Your task to perform on an android device: What's the news in India? Image 0: 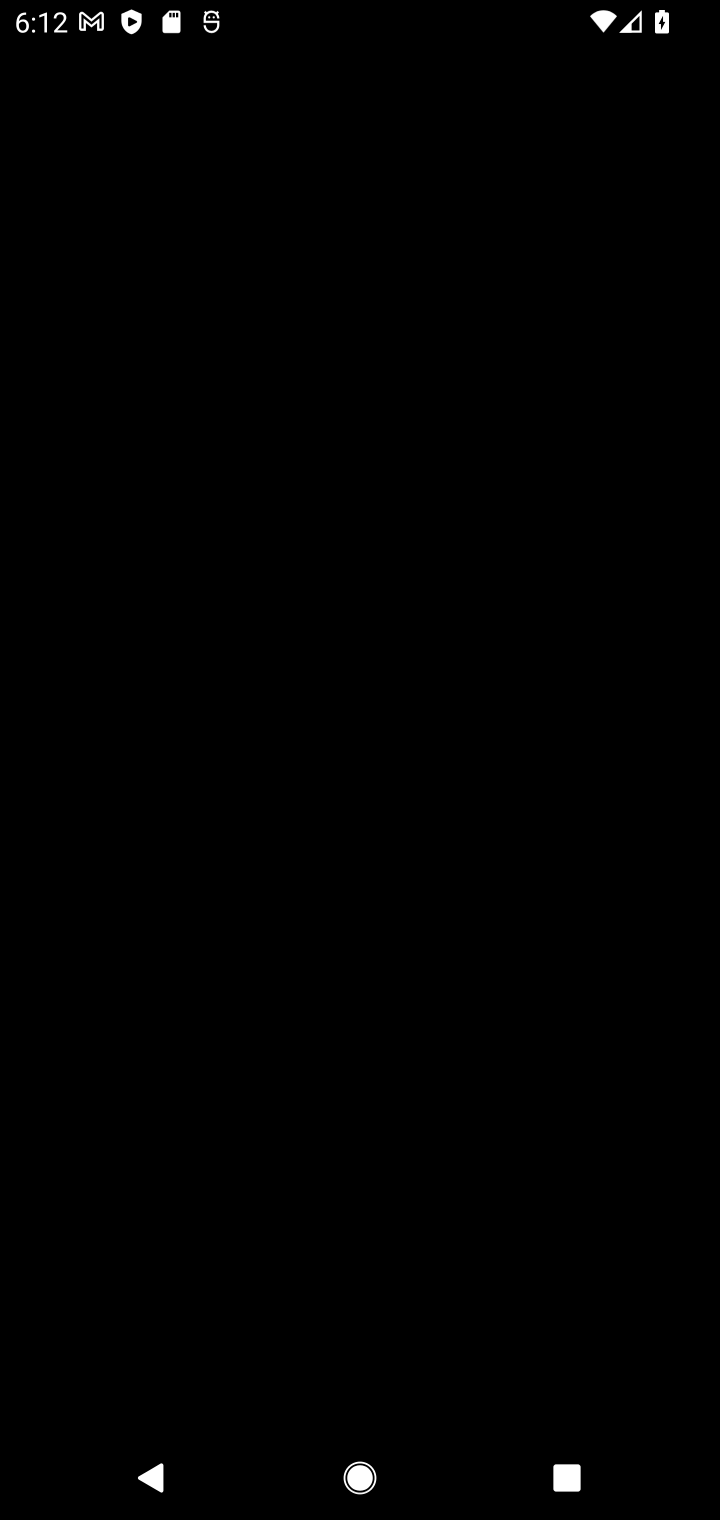
Step 0: press home button
Your task to perform on an android device: What's the news in India? Image 1: 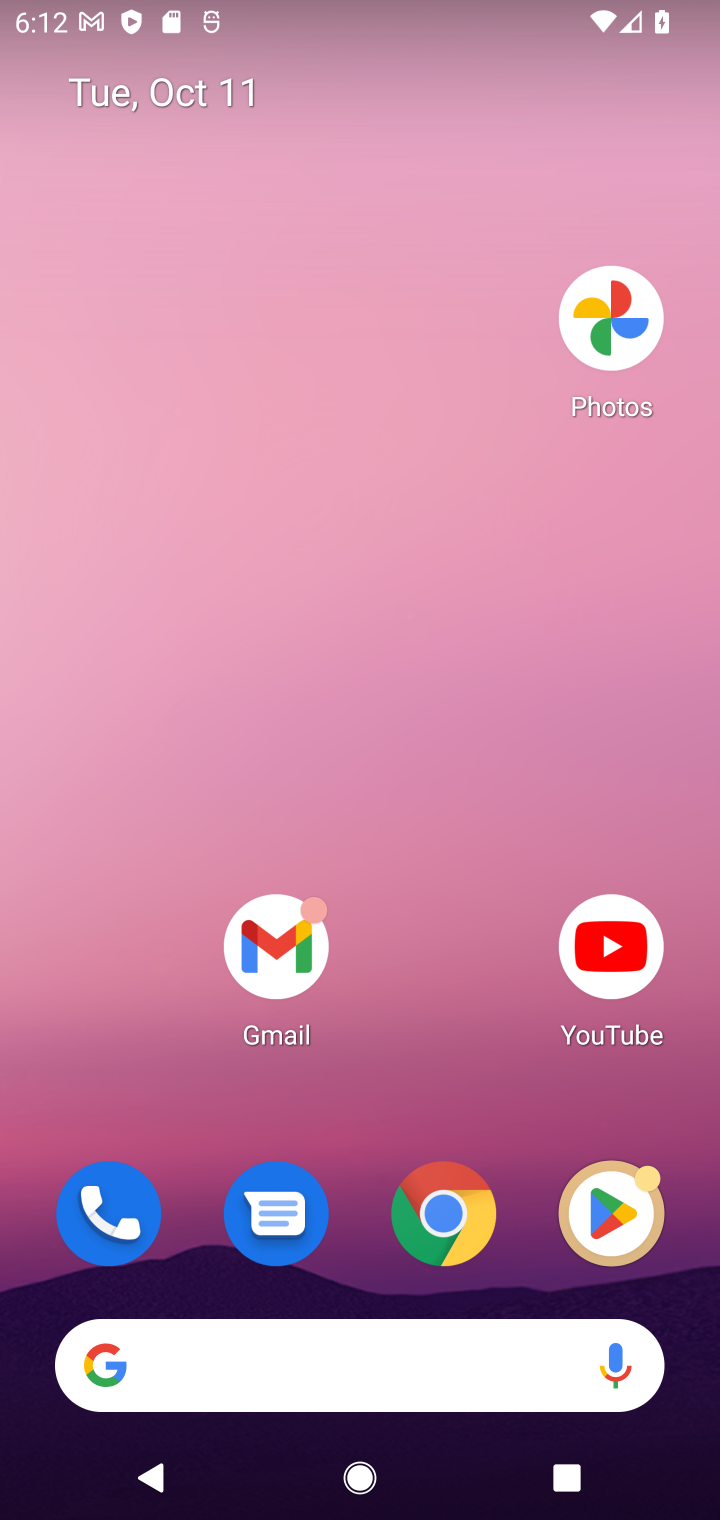
Step 1: drag from (382, 1139) to (526, 72)
Your task to perform on an android device: What's the news in India? Image 2: 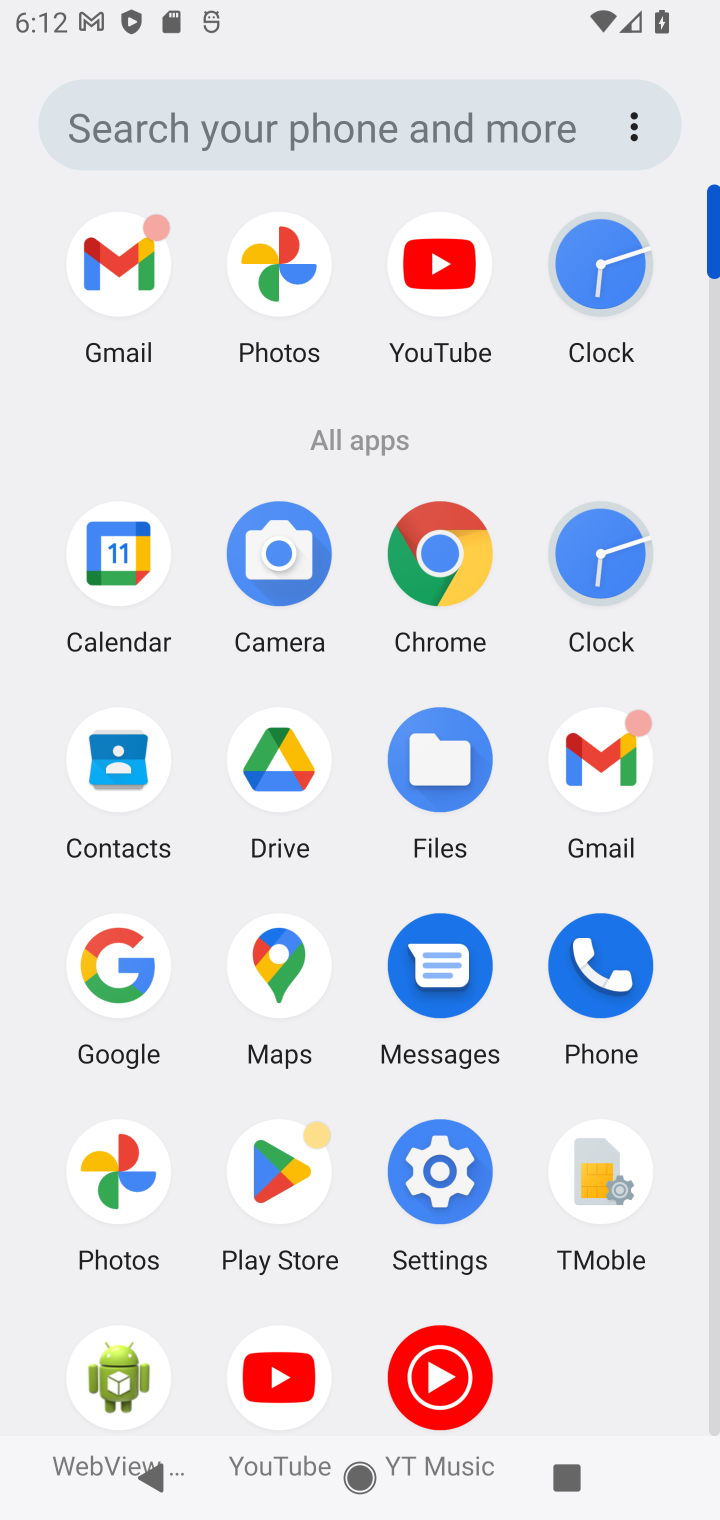
Step 2: click (441, 554)
Your task to perform on an android device: What's the news in India? Image 3: 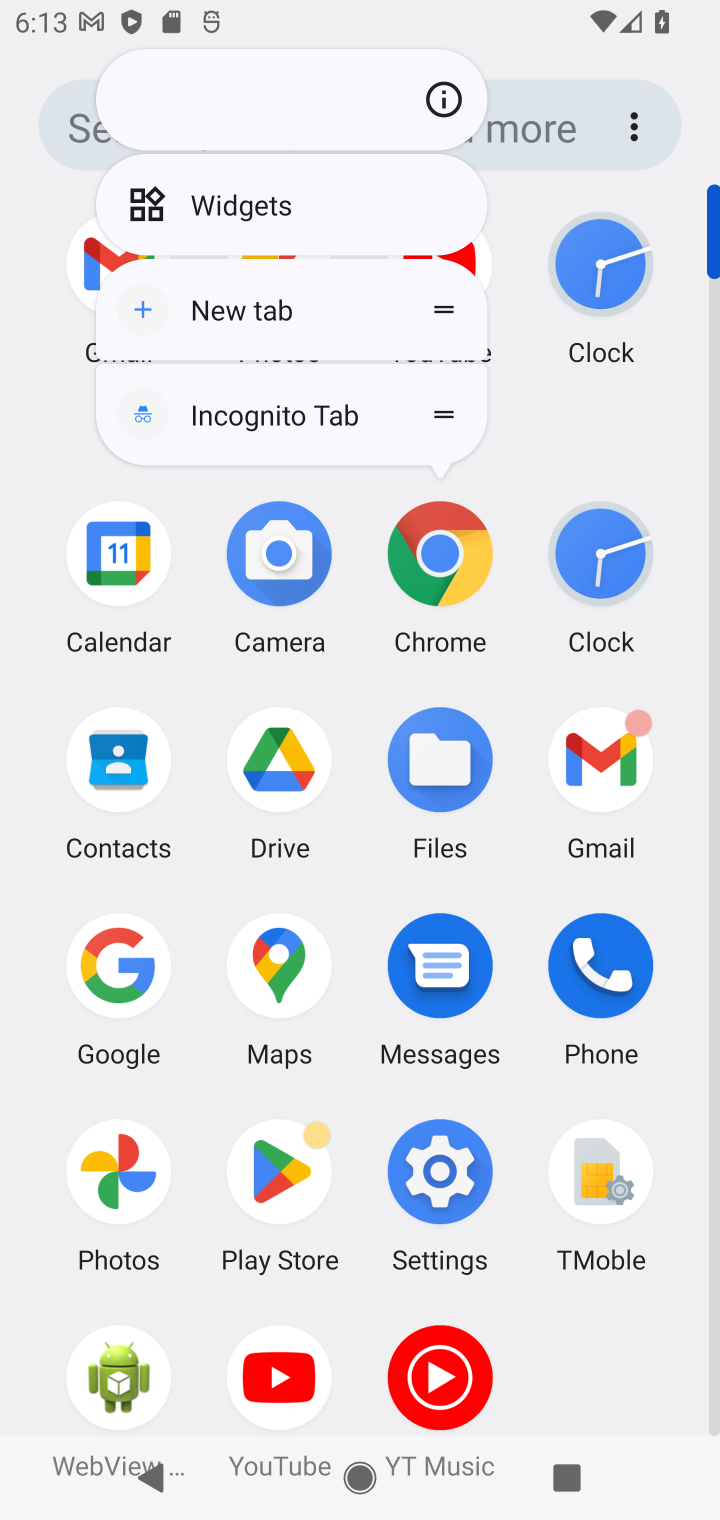
Step 3: click (436, 572)
Your task to perform on an android device: What's the news in India? Image 4: 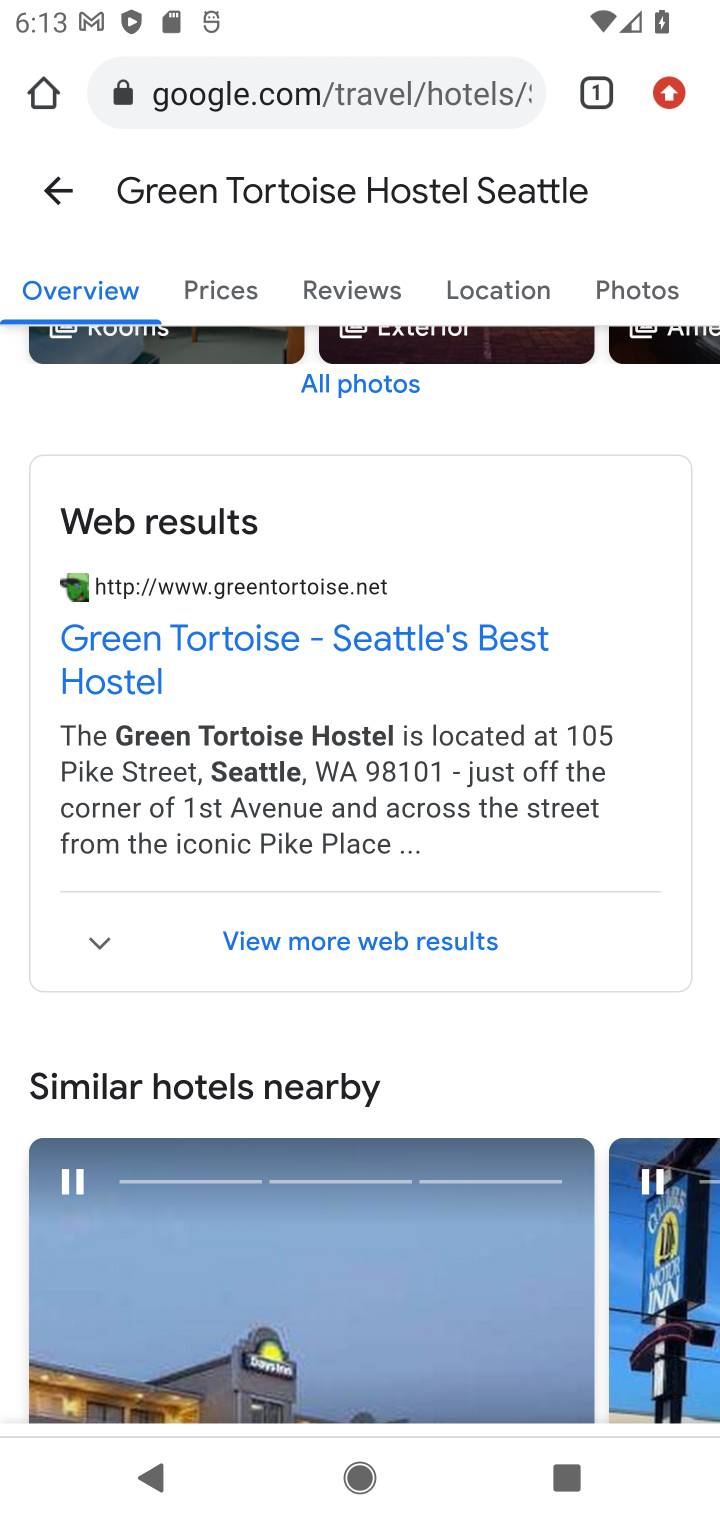
Step 4: click (378, 83)
Your task to perform on an android device: What's the news in India? Image 5: 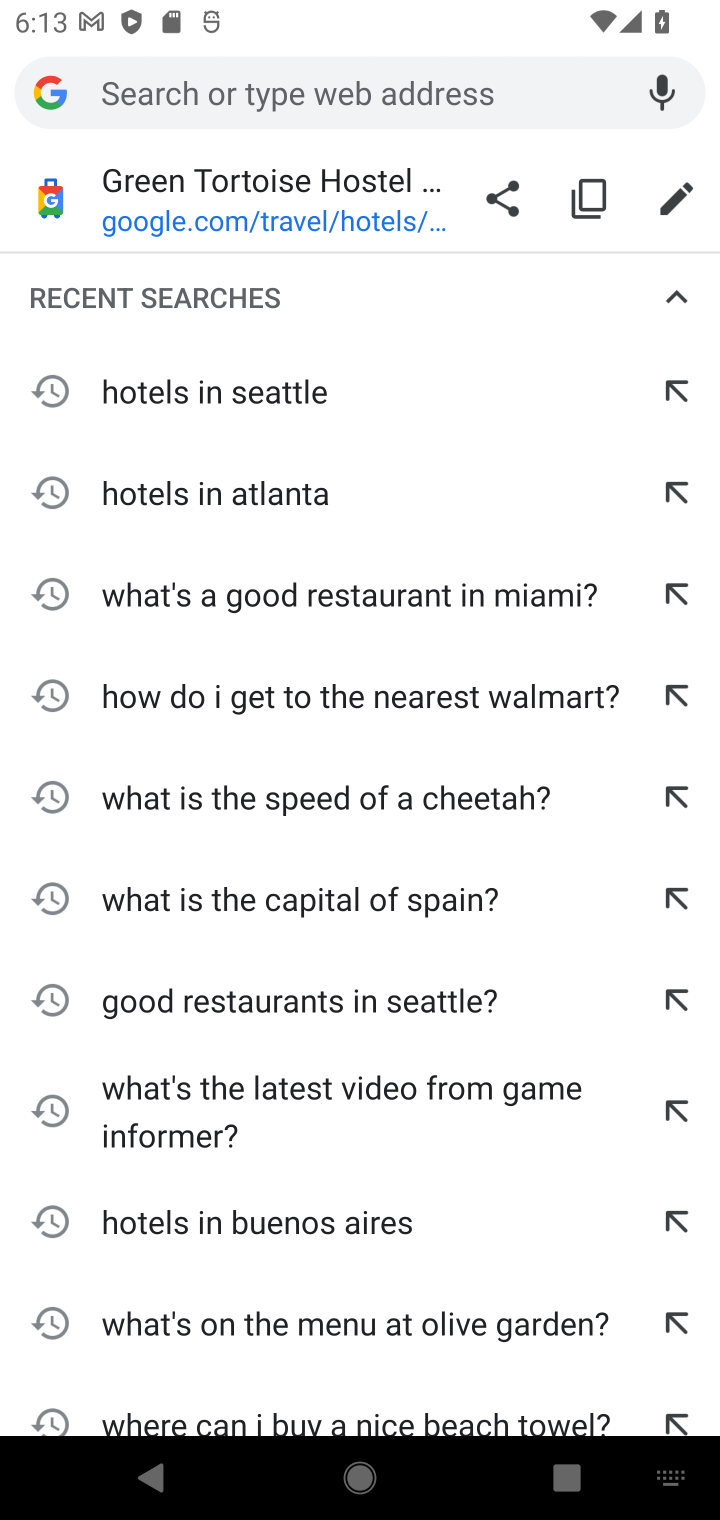
Step 5: type "hotels in Seattle"
Your task to perform on an android device: What's the news in India? Image 6: 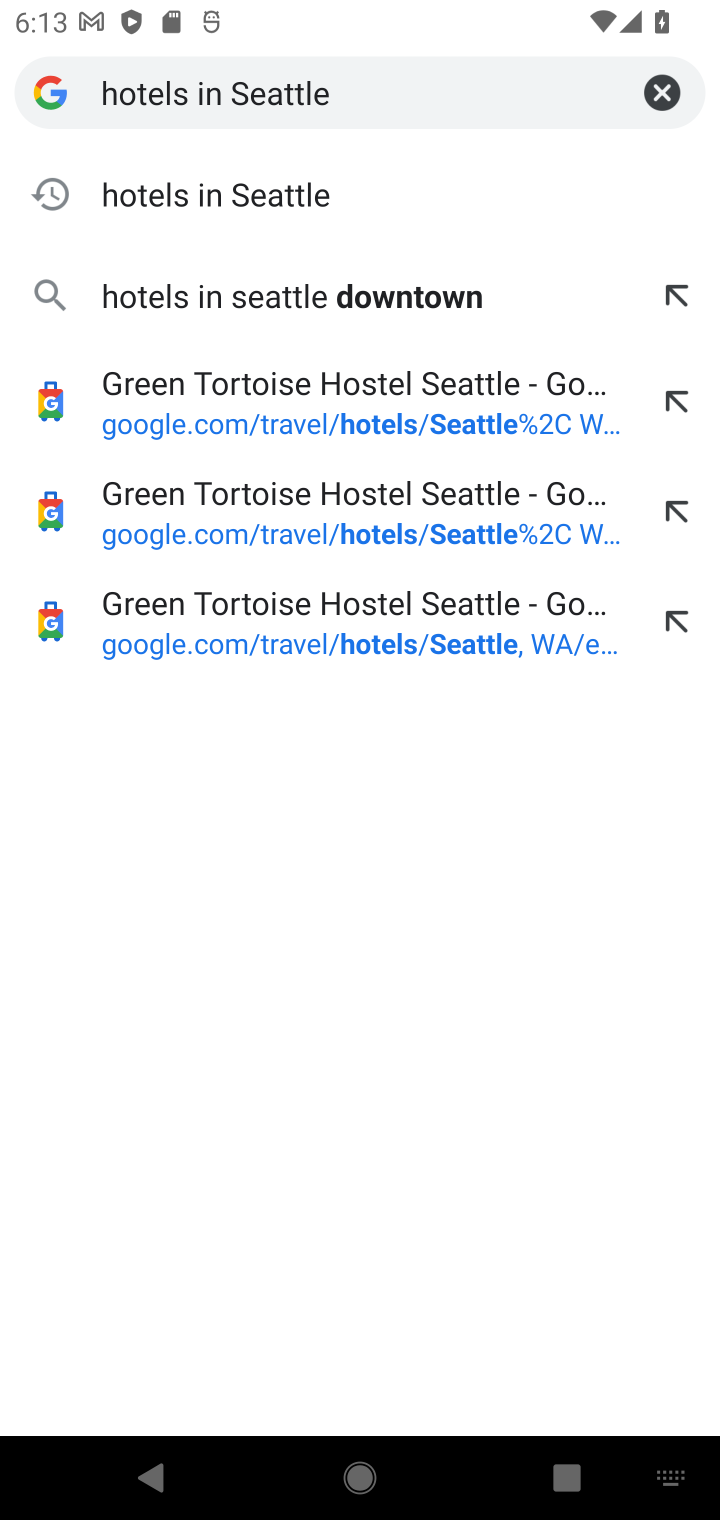
Step 6: press enter
Your task to perform on an android device: What's the news in India? Image 7: 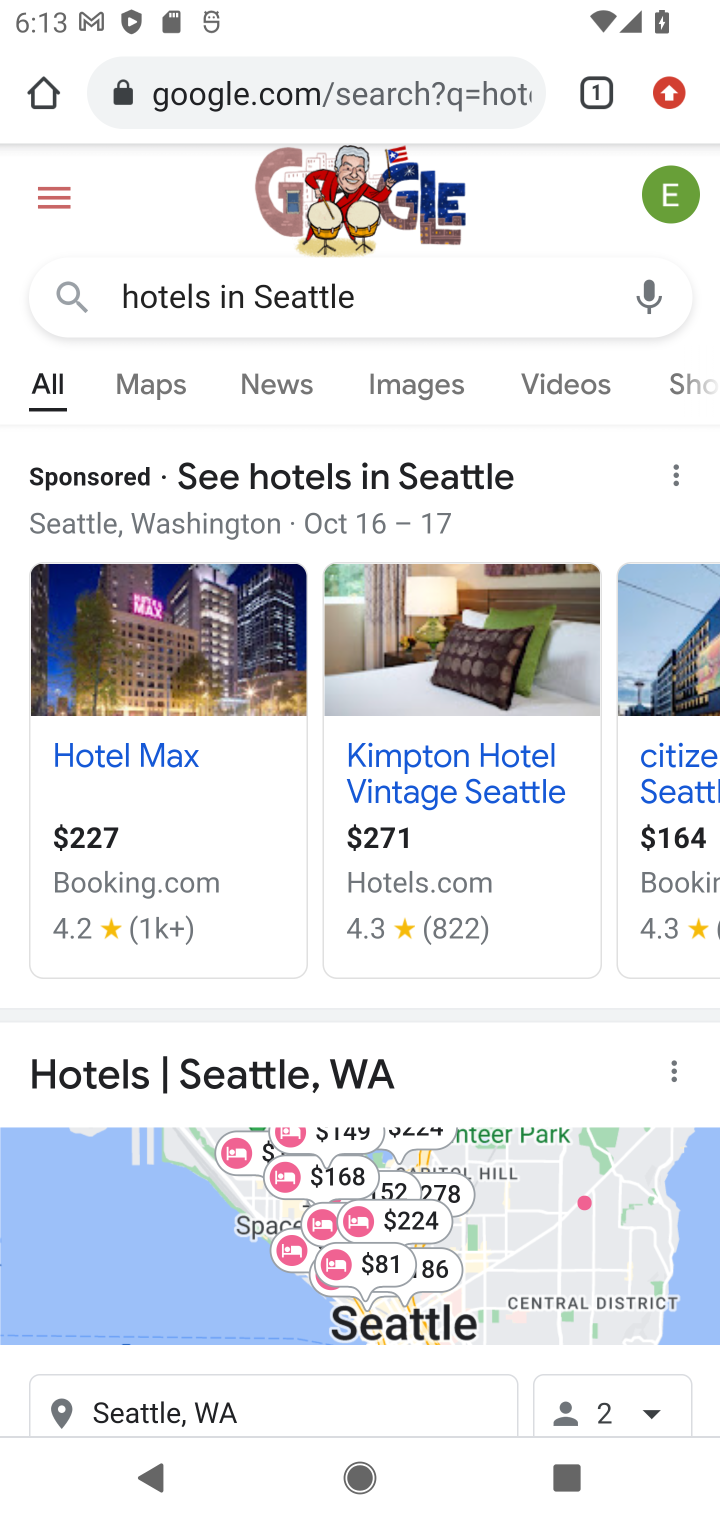
Step 7: click (491, 89)
Your task to perform on an android device: What's the news in India? Image 8: 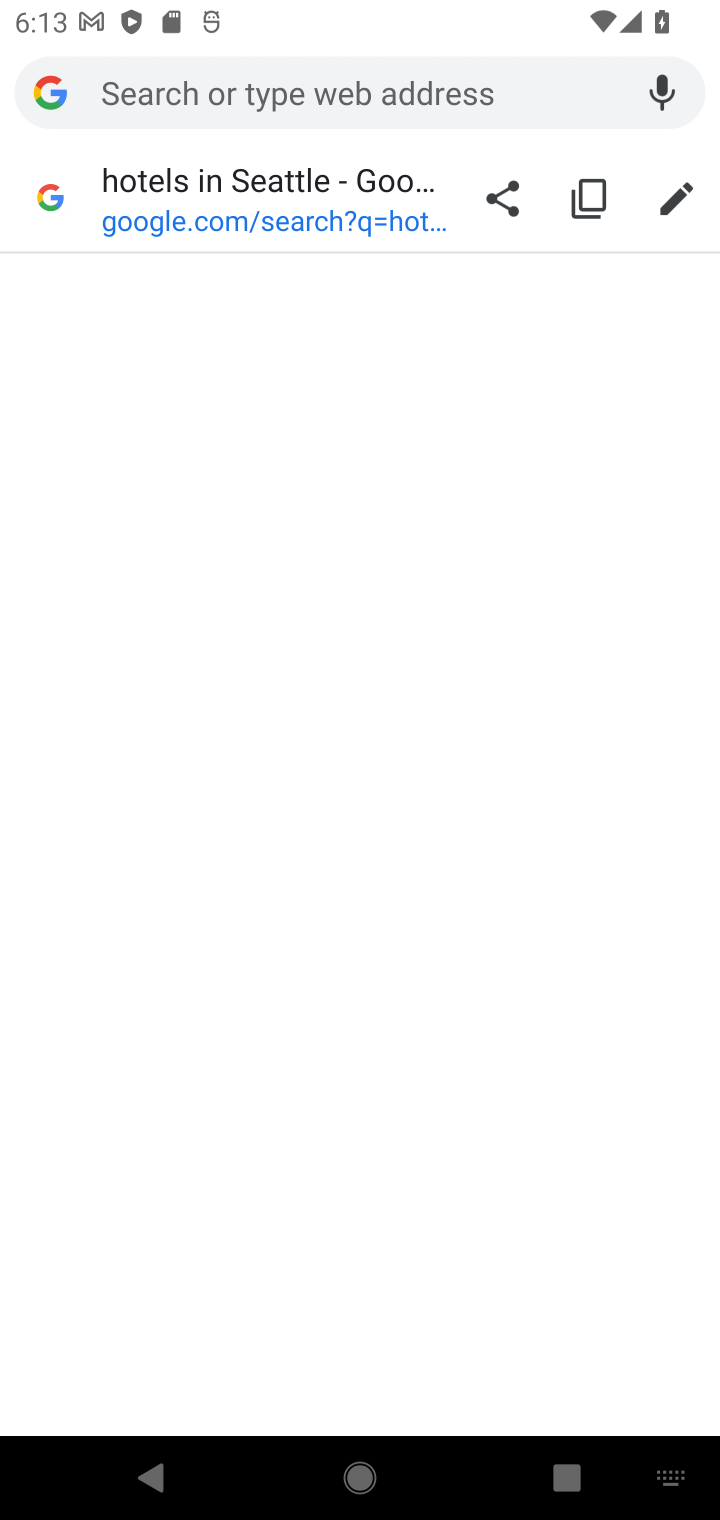
Step 8: type "What's the news in India?"
Your task to perform on an android device: What's the news in India? Image 9: 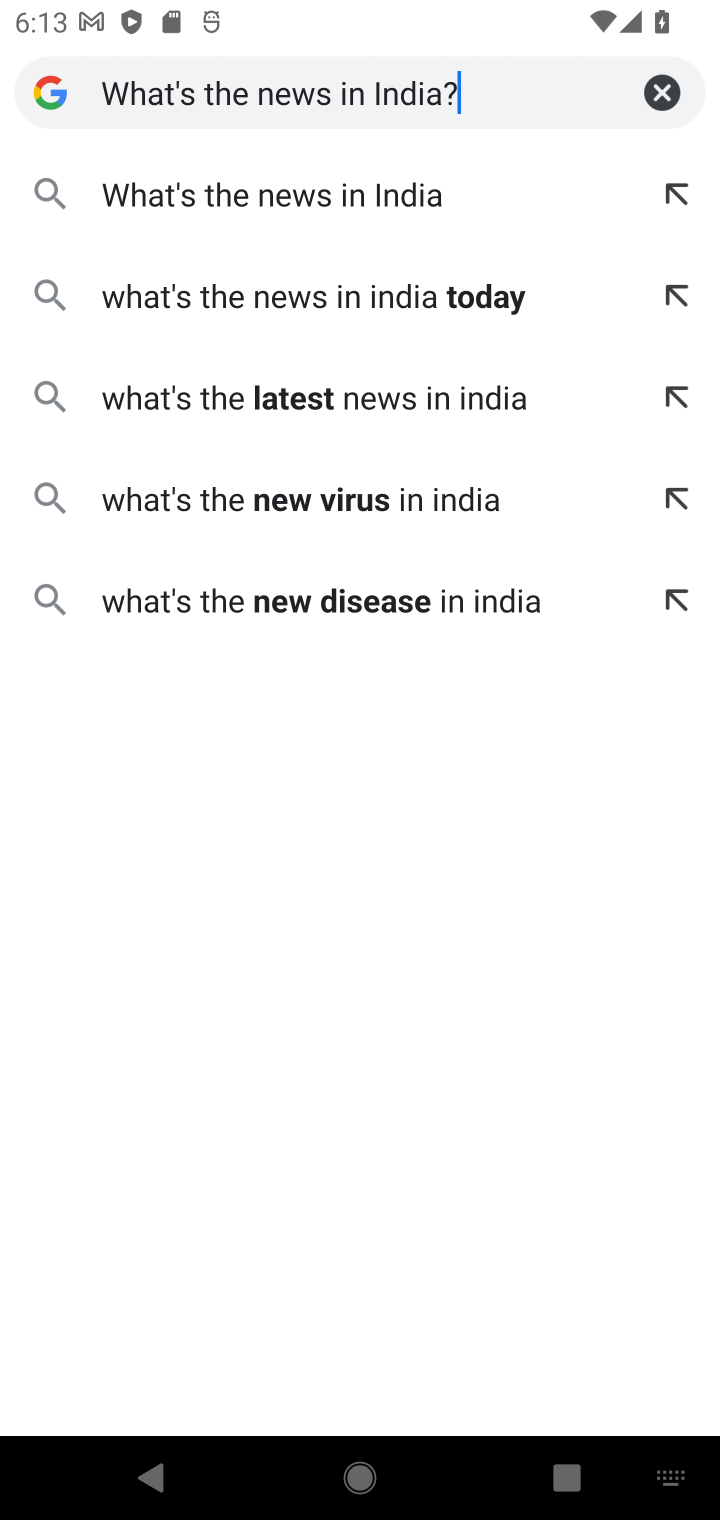
Step 9: type ""
Your task to perform on an android device: What's the news in India? Image 10: 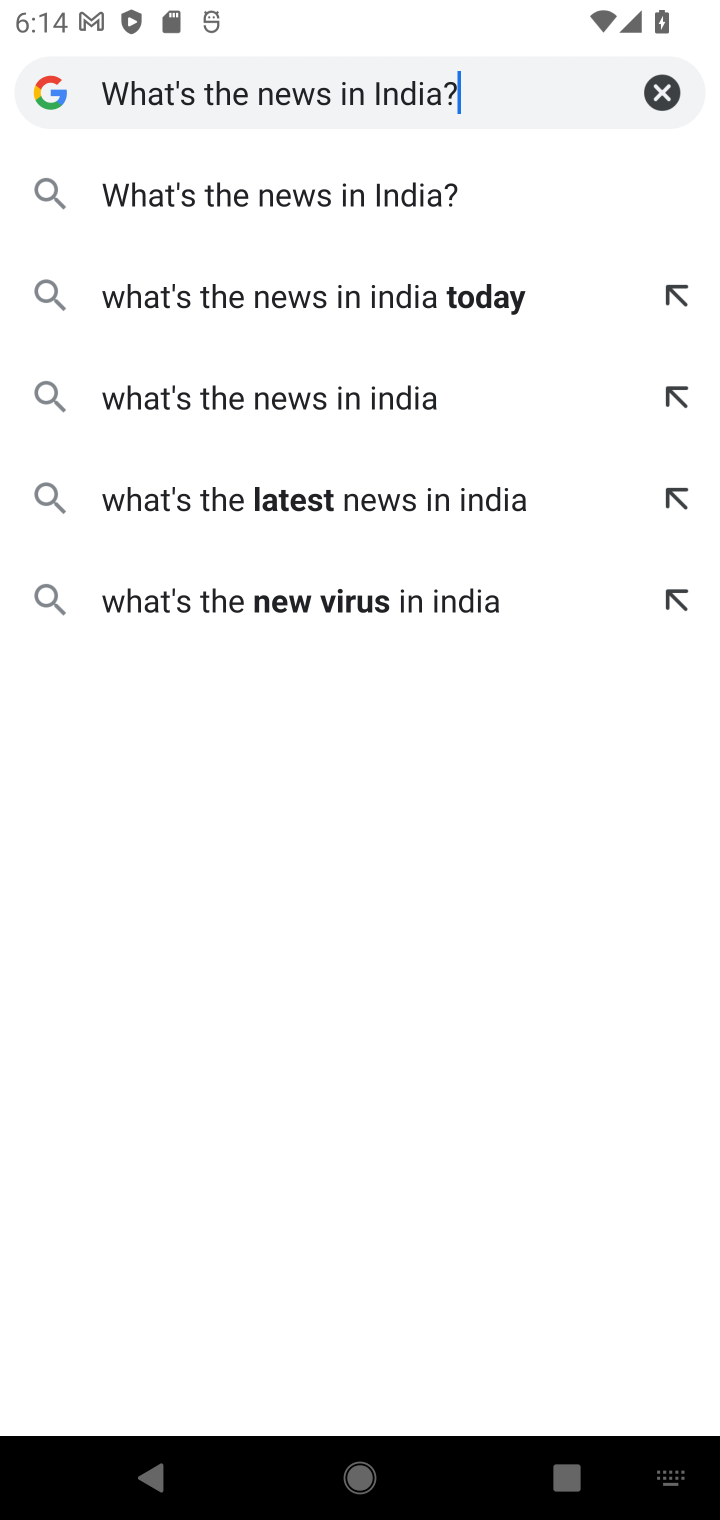
Step 10: click (334, 223)
Your task to perform on an android device: What's the news in India? Image 11: 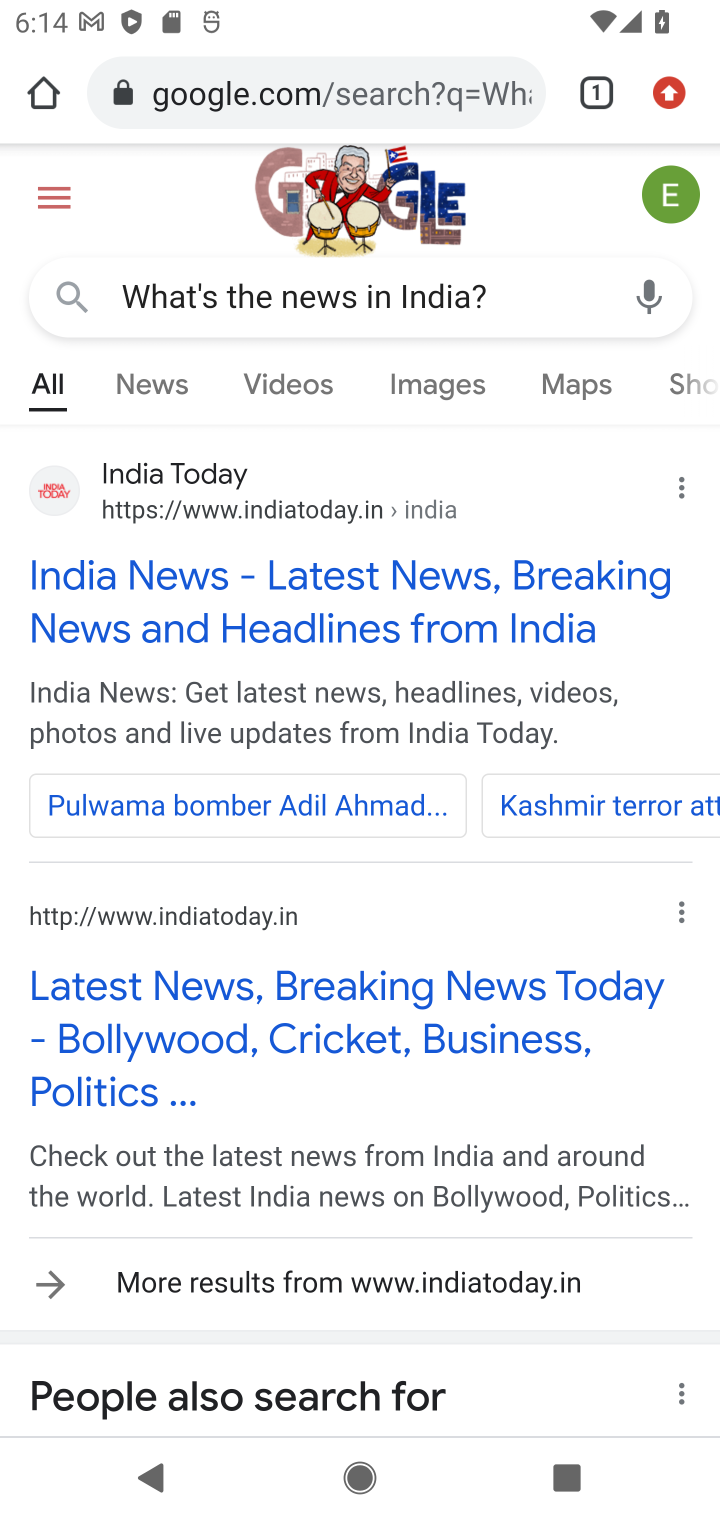
Step 11: click (173, 585)
Your task to perform on an android device: What's the news in India? Image 12: 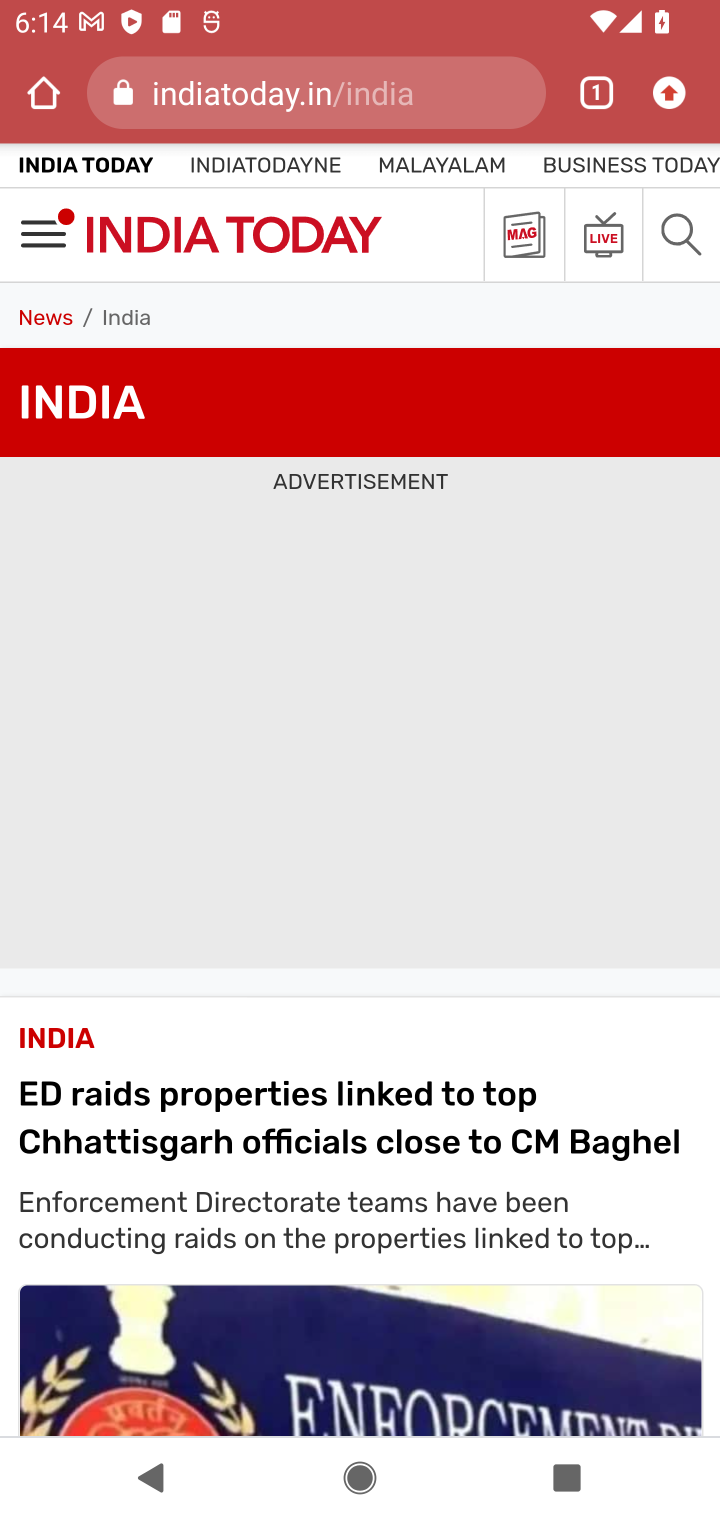
Step 12: drag from (153, 1277) to (125, 456)
Your task to perform on an android device: What's the news in India? Image 13: 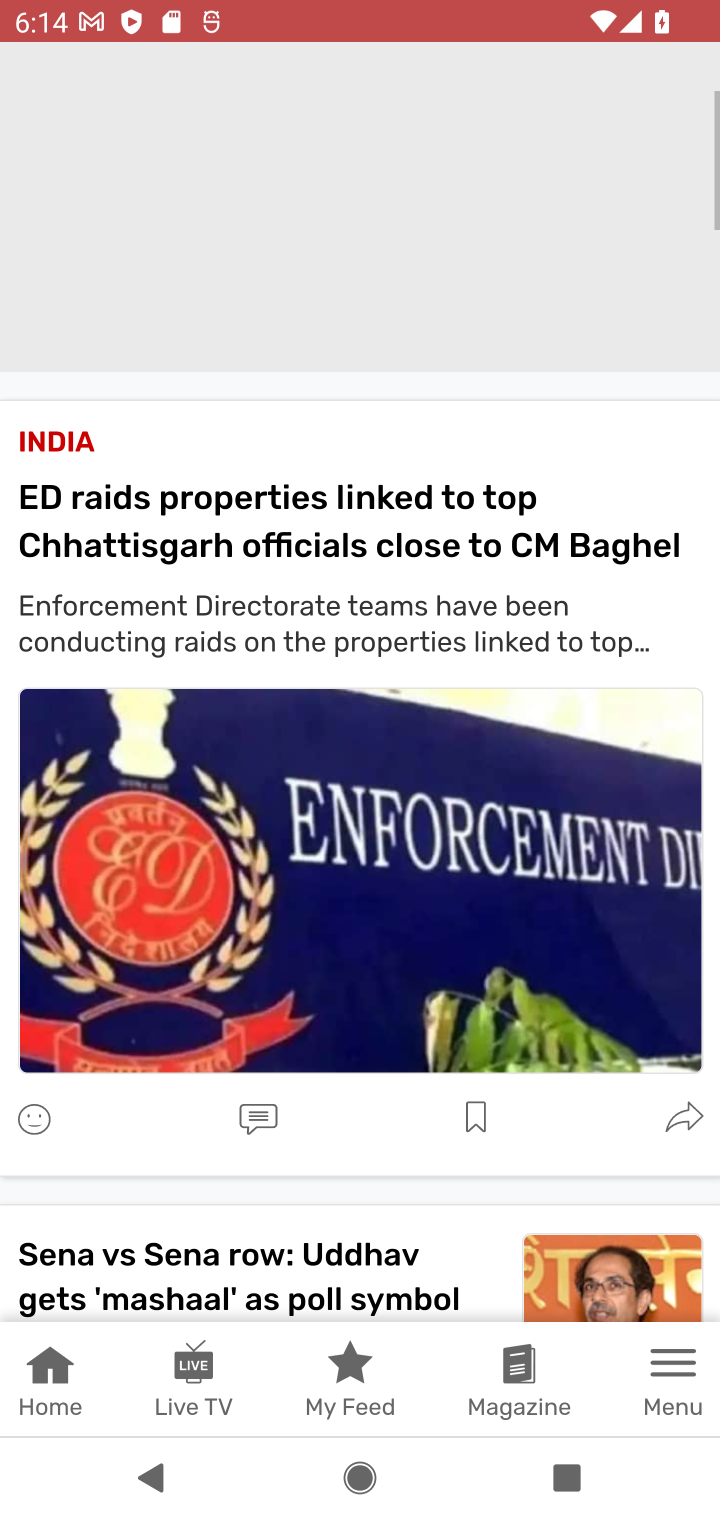
Step 13: drag from (282, 956) to (359, 257)
Your task to perform on an android device: What's the news in India? Image 14: 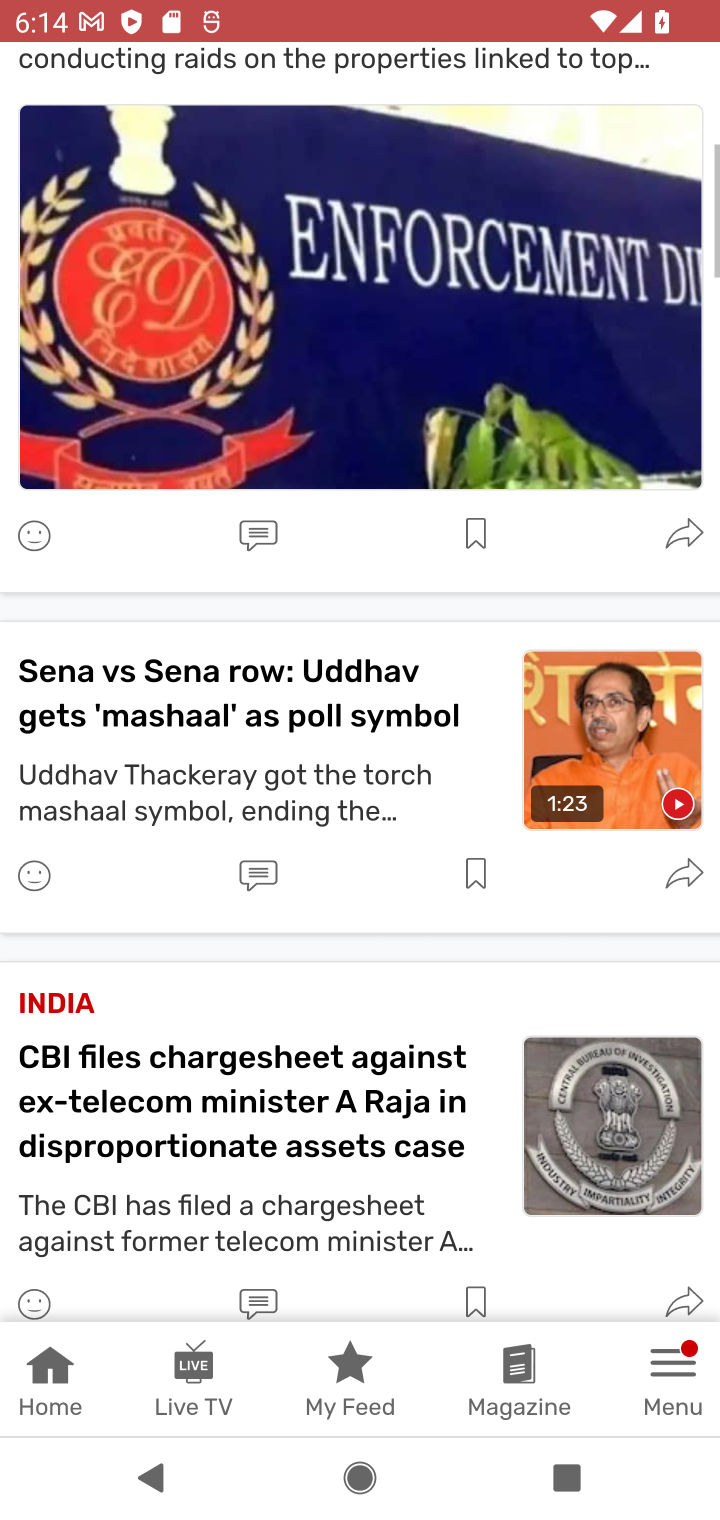
Step 14: drag from (207, 1140) to (285, 21)
Your task to perform on an android device: What's the news in India? Image 15: 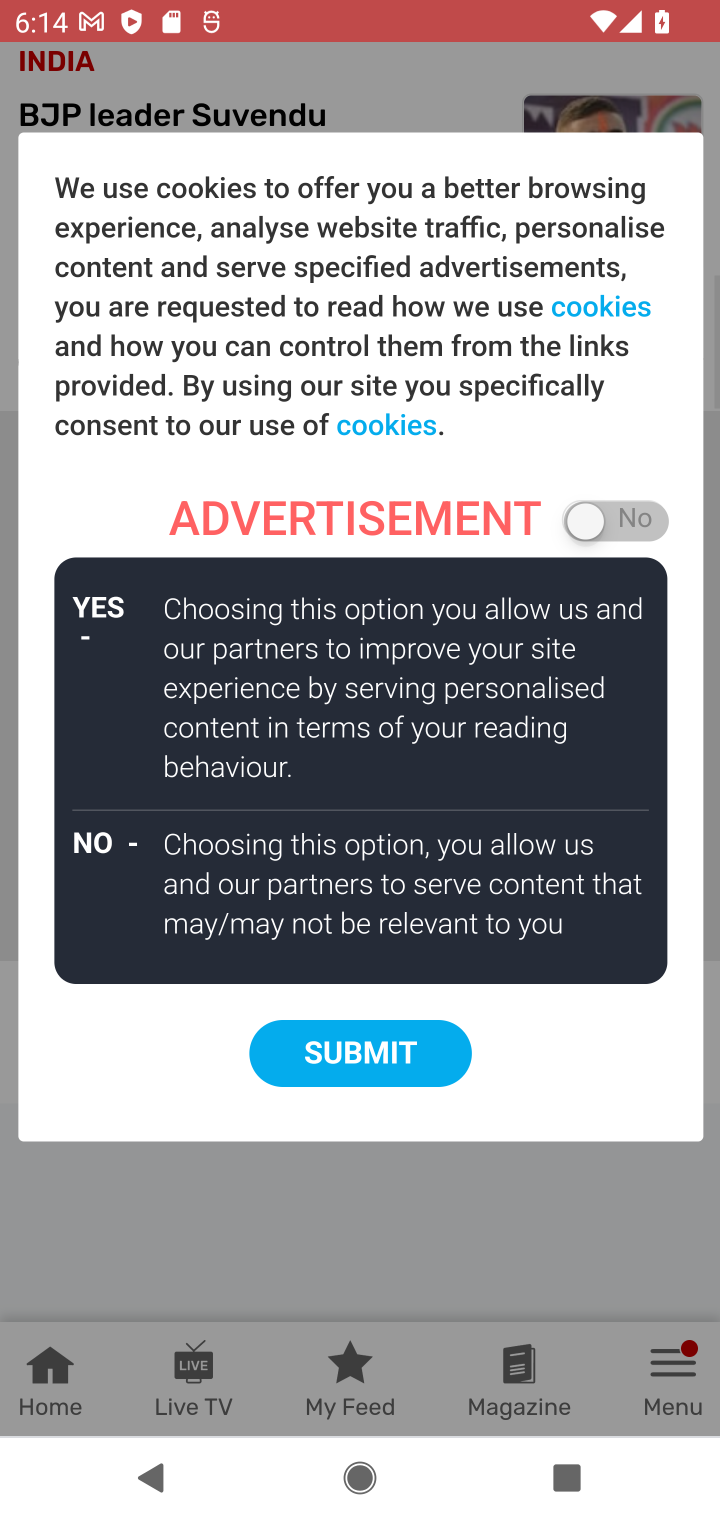
Step 15: drag from (229, 1002) to (223, 136)
Your task to perform on an android device: What's the news in India? Image 16: 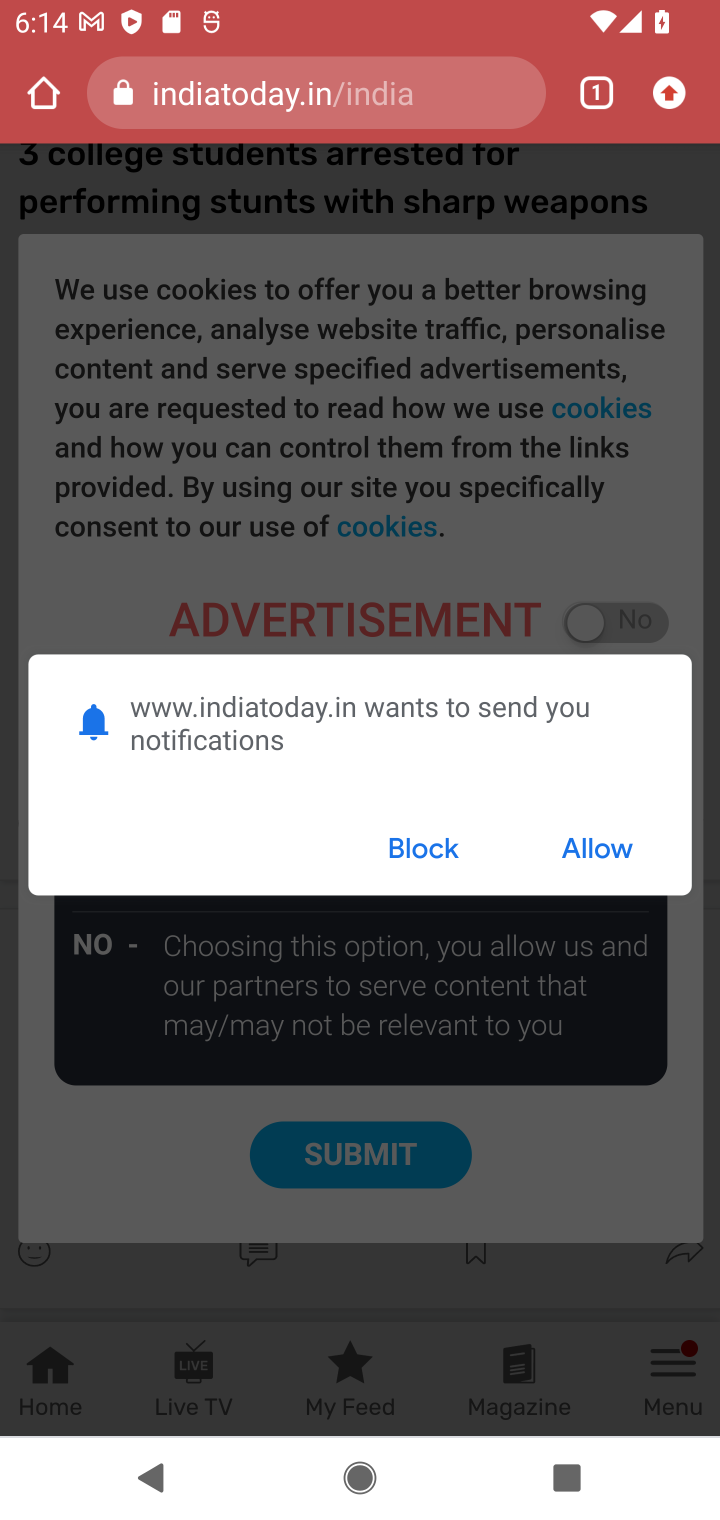
Step 16: click (449, 830)
Your task to perform on an android device: What's the news in India? Image 17: 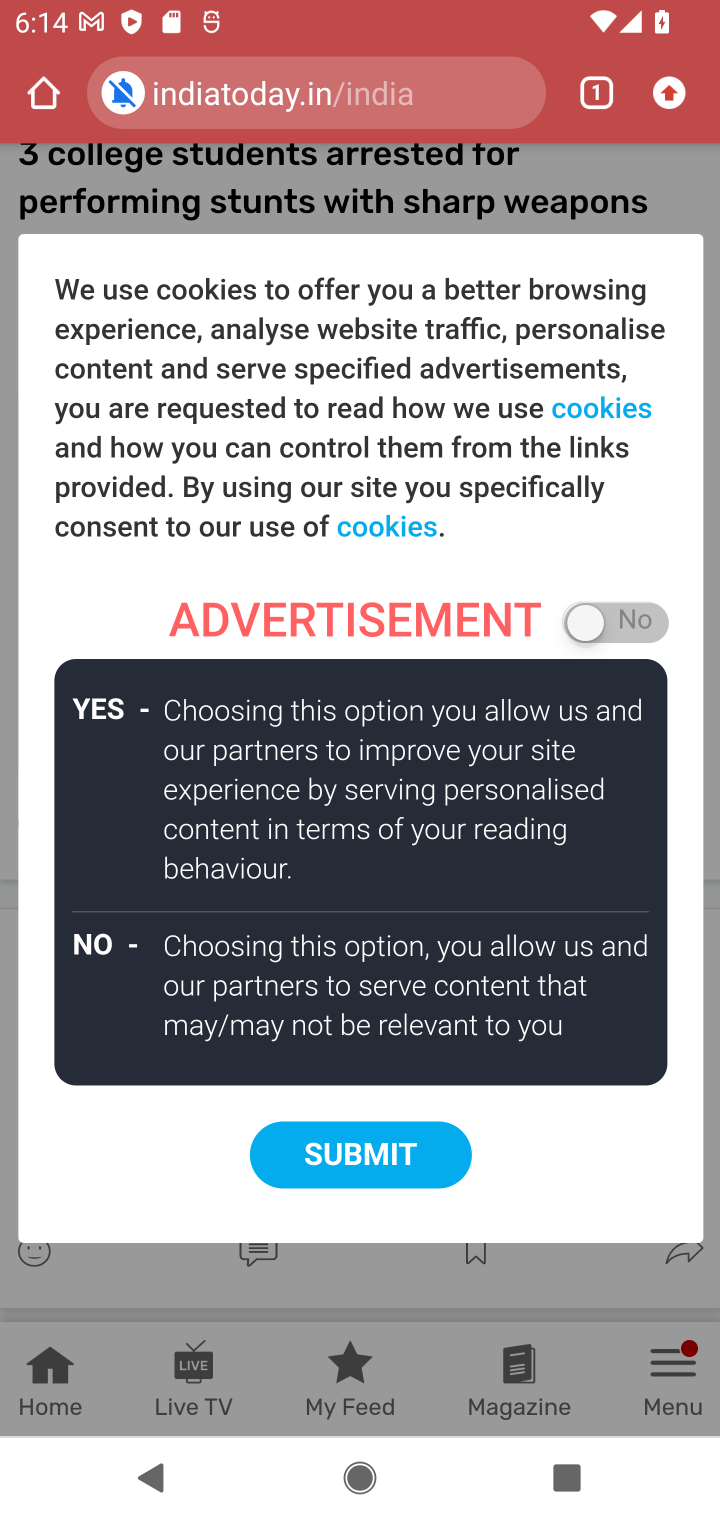
Step 17: click (367, 1151)
Your task to perform on an android device: What's the news in India? Image 18: 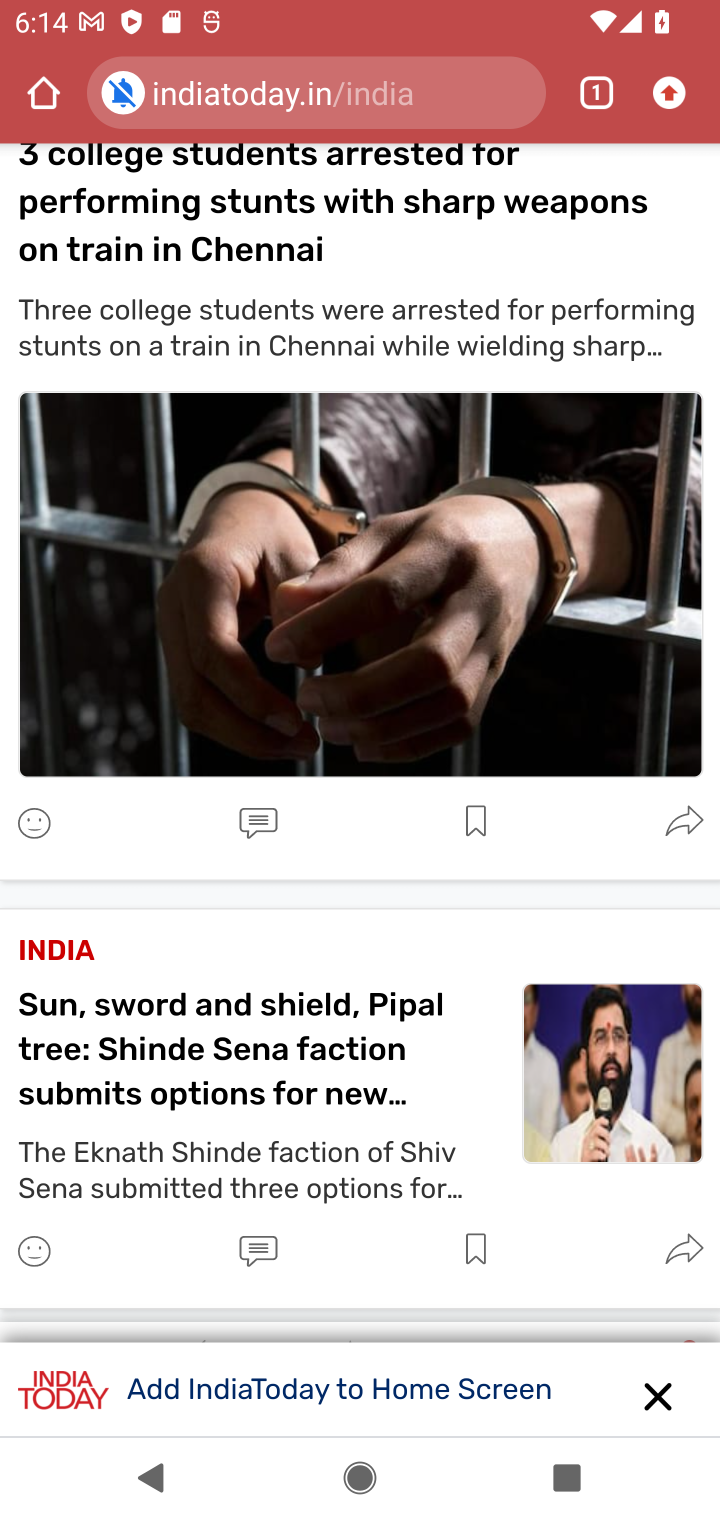
Step 18: drag from (390, 818) to (461, 434)
Your task to perform on an android device: What's the news in India? Image 19: 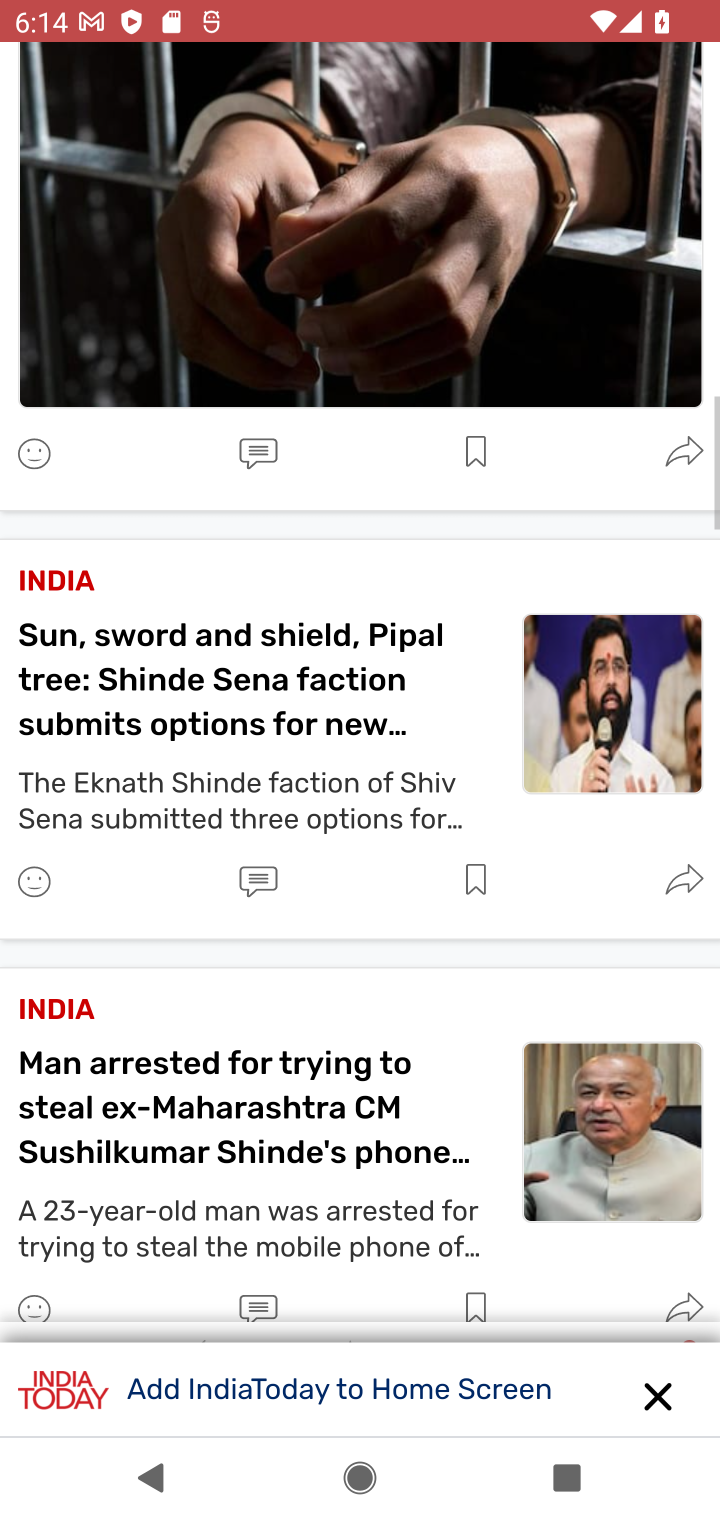
Step 19: drag from (458, 660) to (491, 281)
Your task to perform on an android device: What's the news in India? Image 20: 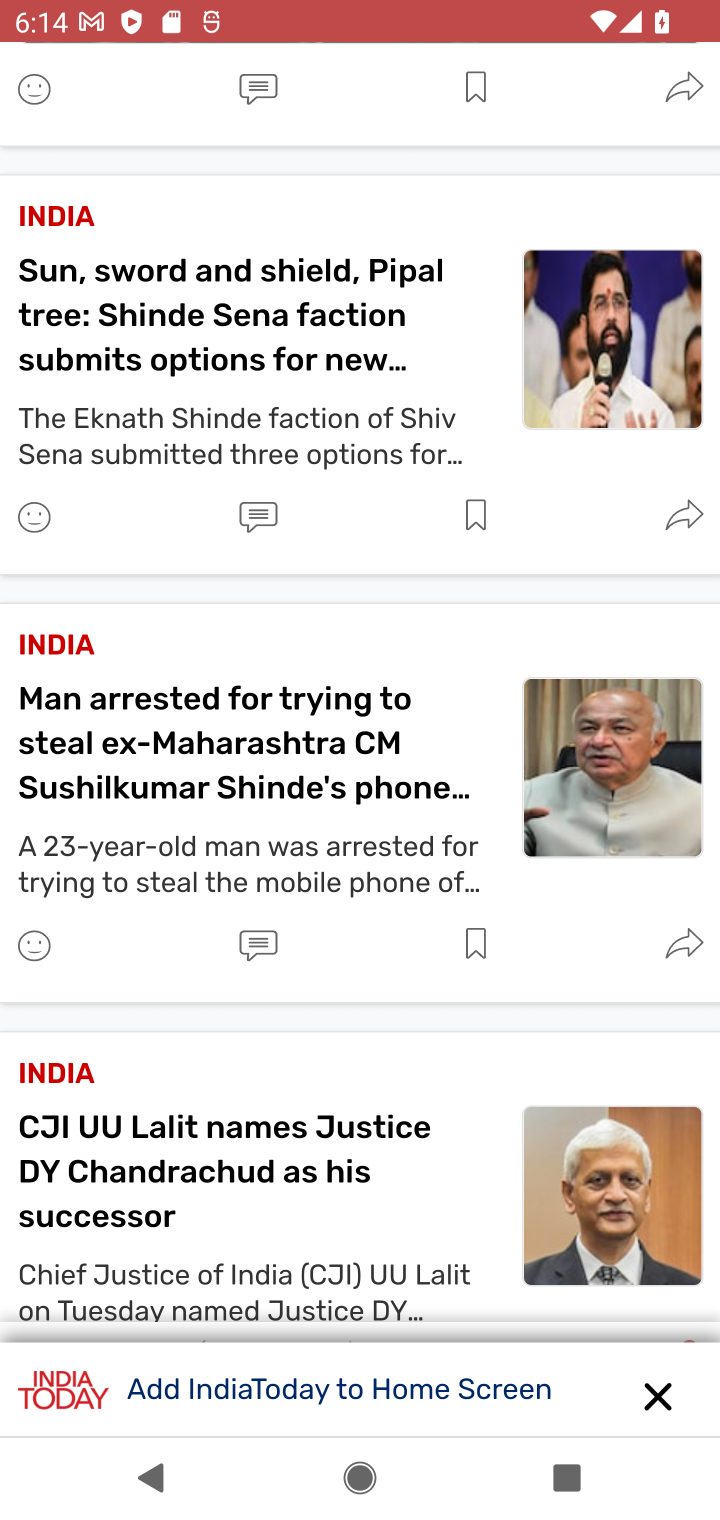
Step 20: drag from (443, 1144) to (454, 578)
Your task to perform on an android device: What's the news in India? Image 21: 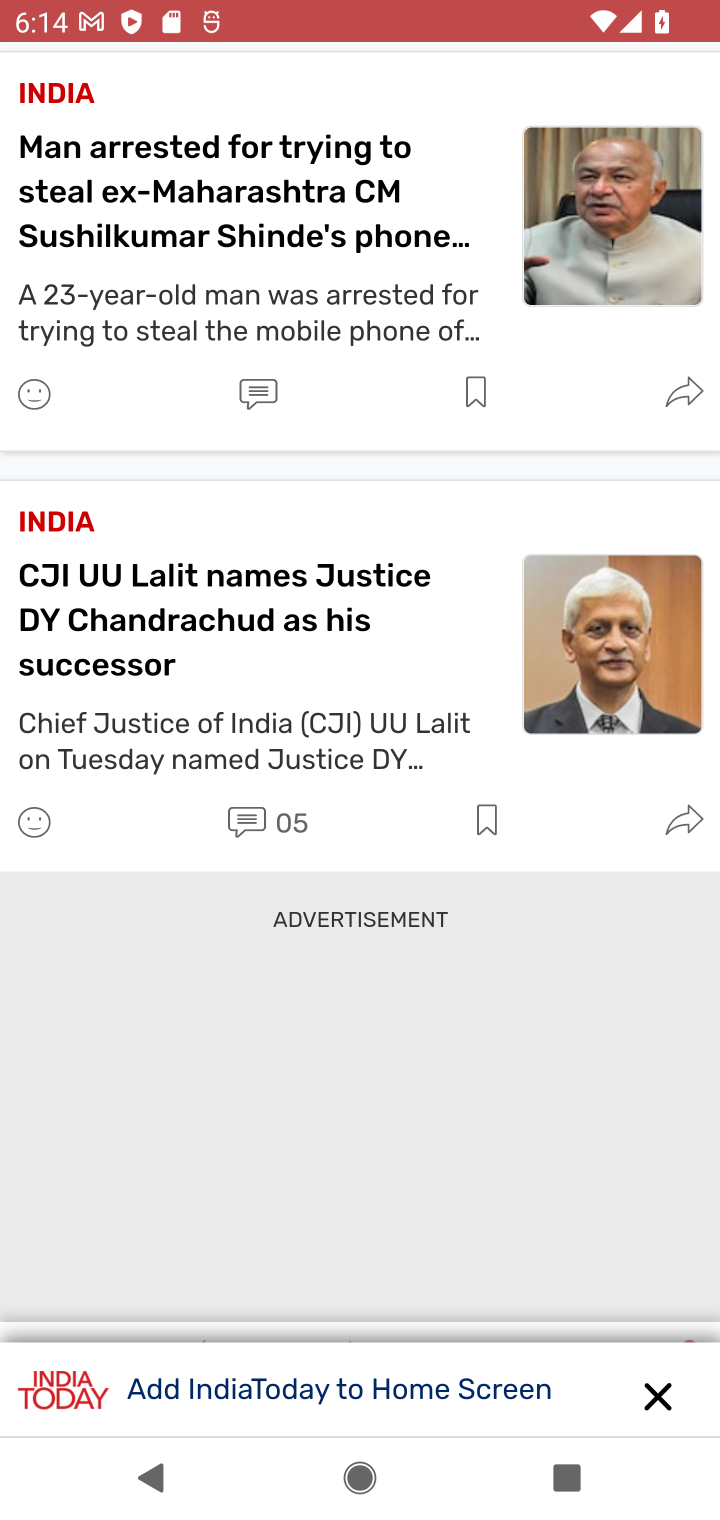
Step 21: drag from (448, 758) to (451, 521)
Your task to perform on an android device: What's the news in India? Image 22: 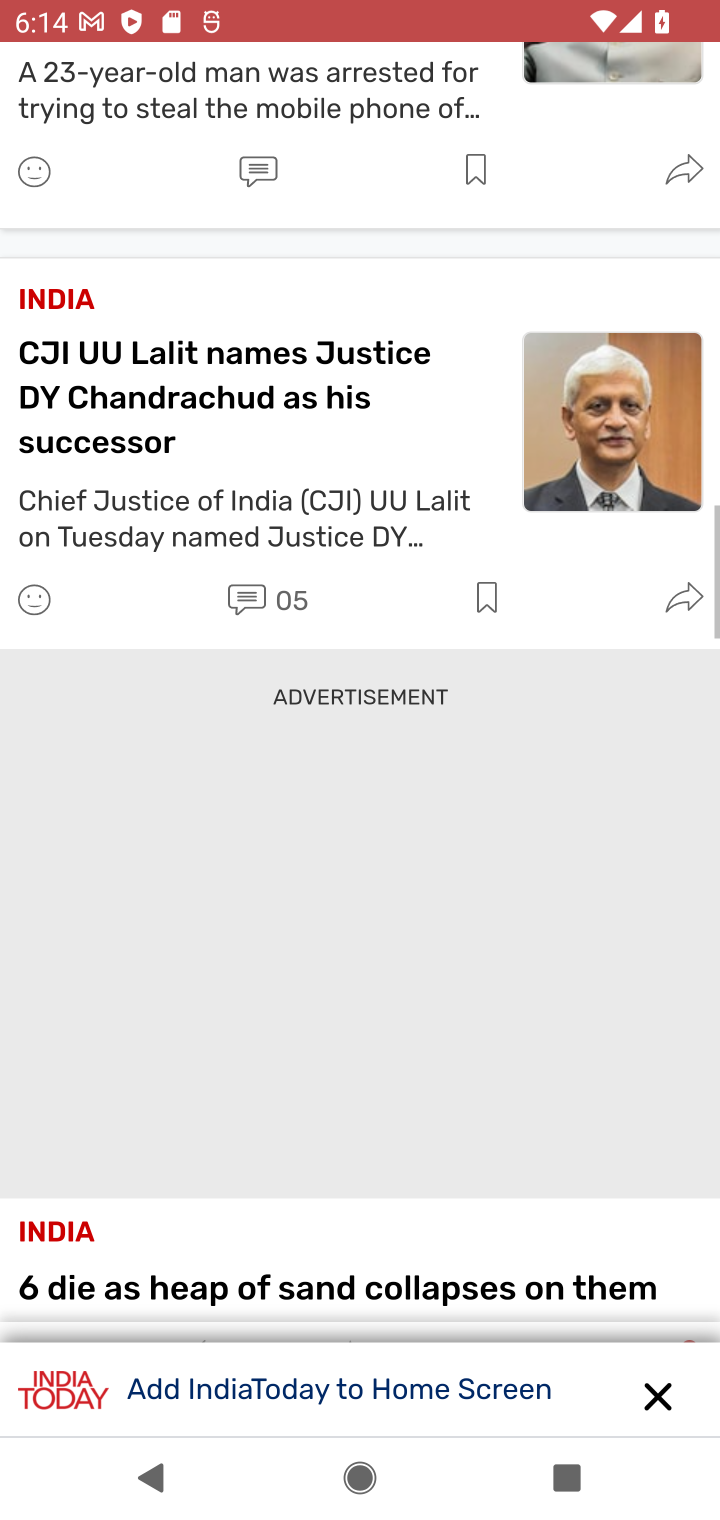
Step 22: press back button
Your task to perform on an android device: What's the news in India? Image 23: 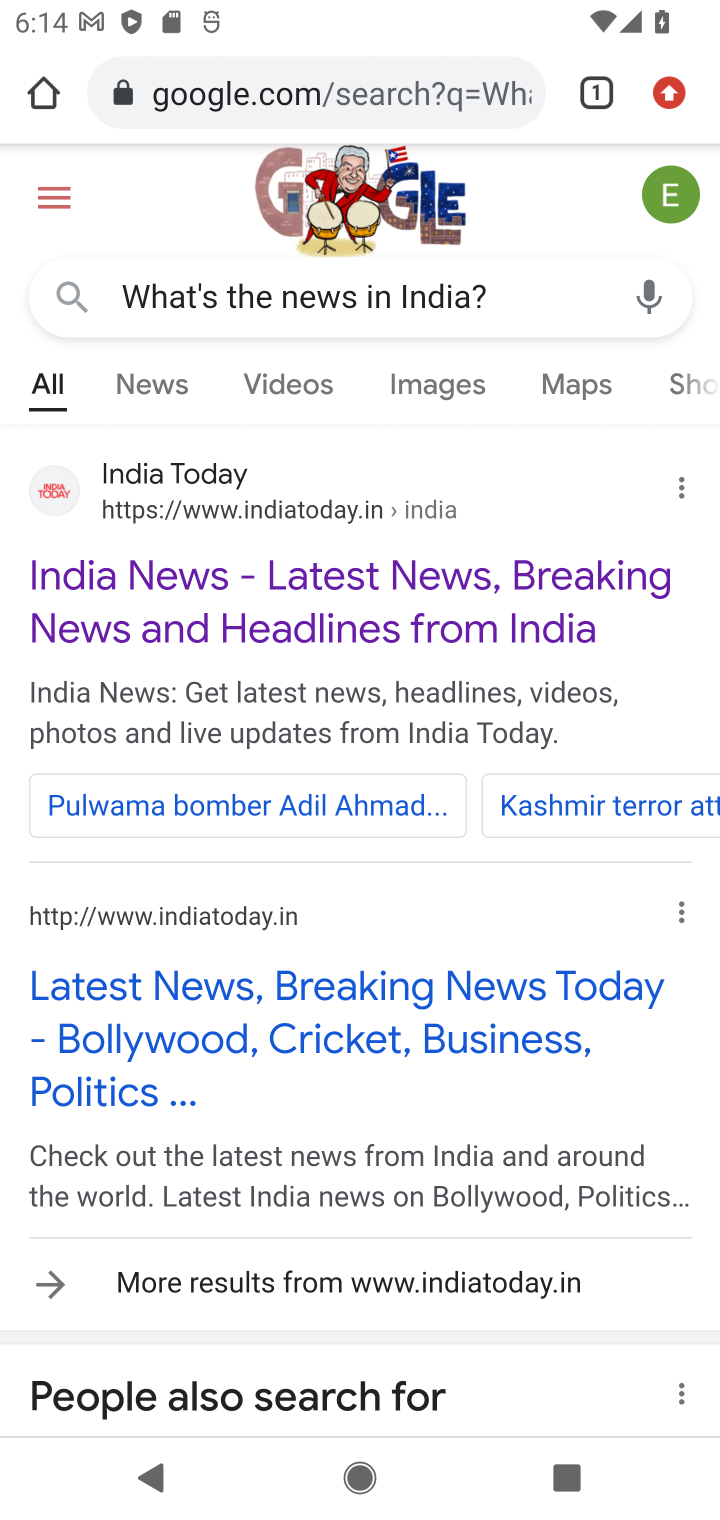
Step 23: drag from (648, 1169) to (637, 583)
Your task to perform on an android device: What's the news in India? Image 24: 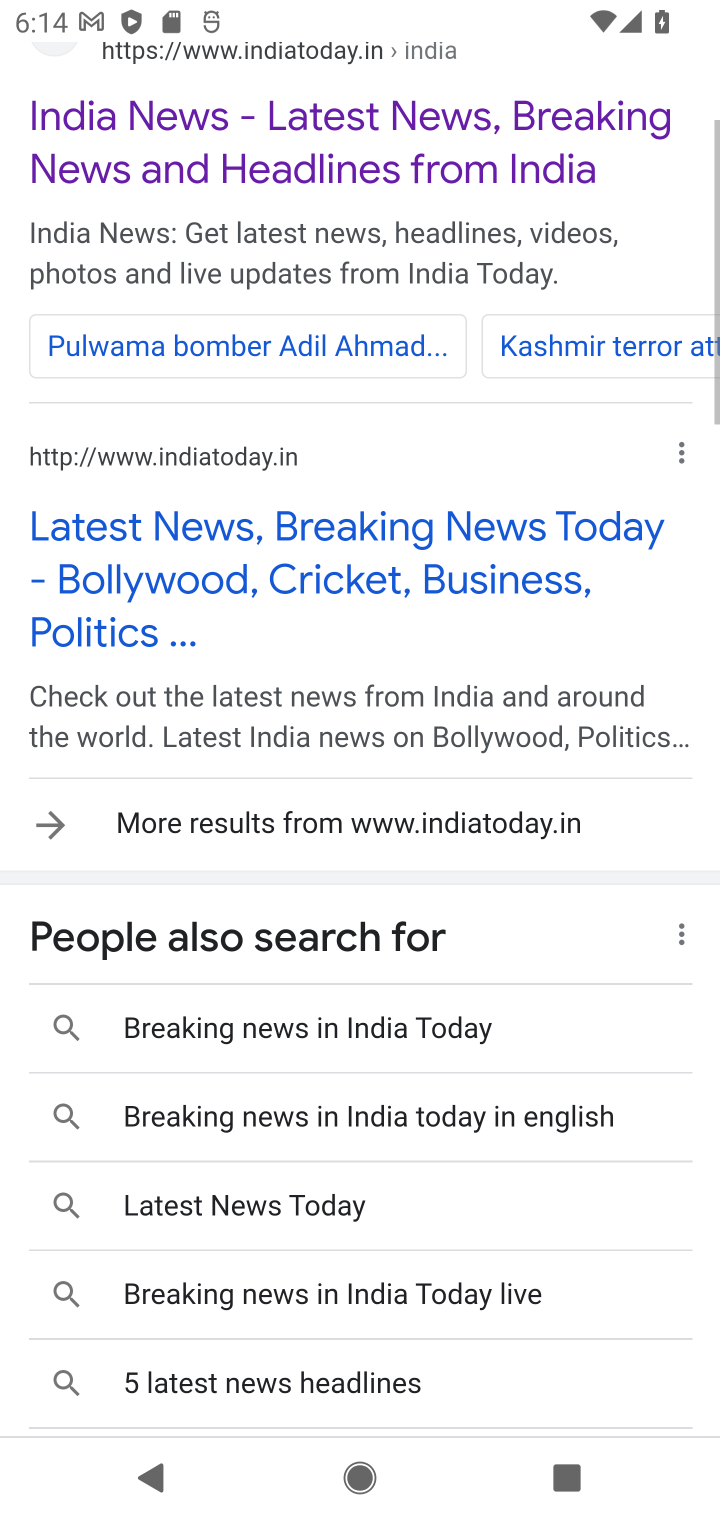
Step 24: click (544, 645)
Your task to perform on an android device: What's the news in India? Image 25: 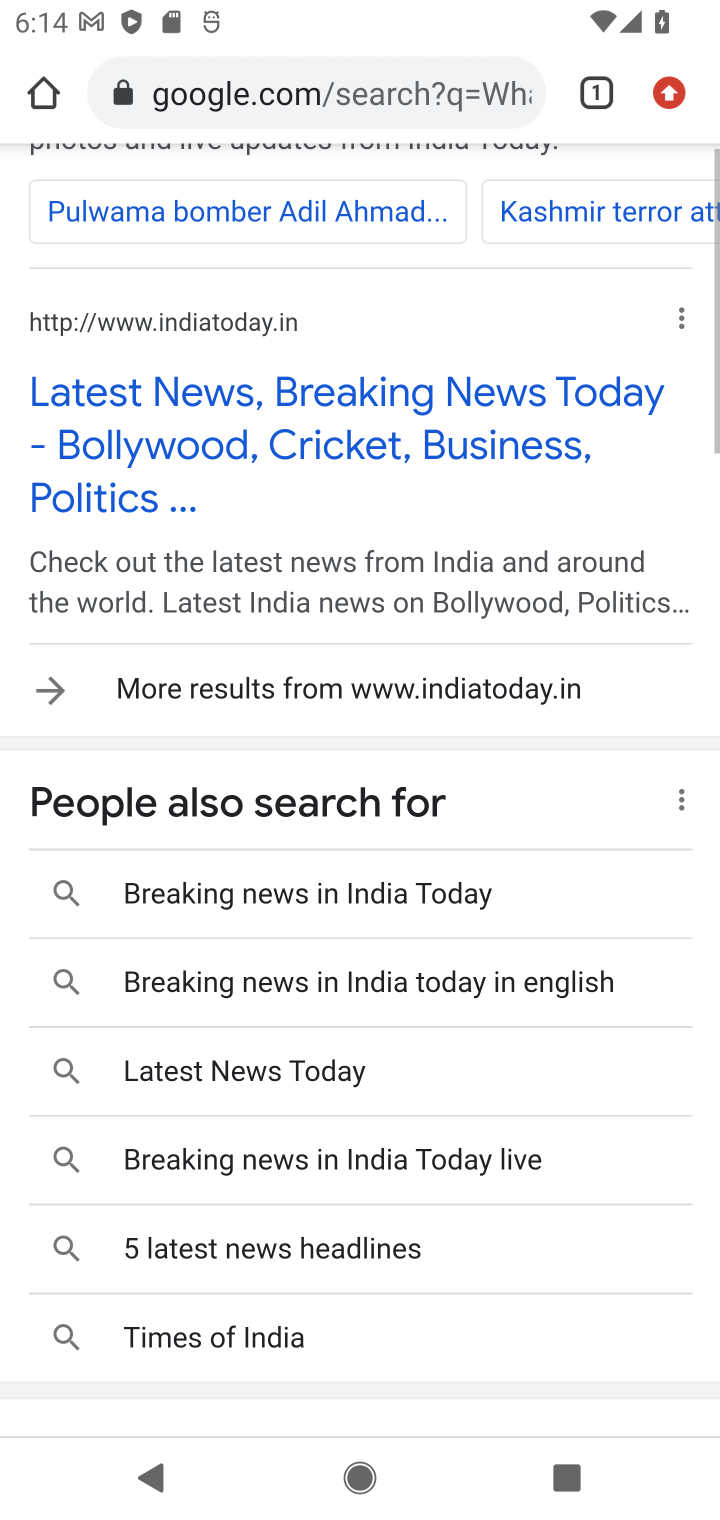
Step 25: drag from (523, 1093) to (528, 639)
Your task to perform on an android device: What's the news in India? Image 26: 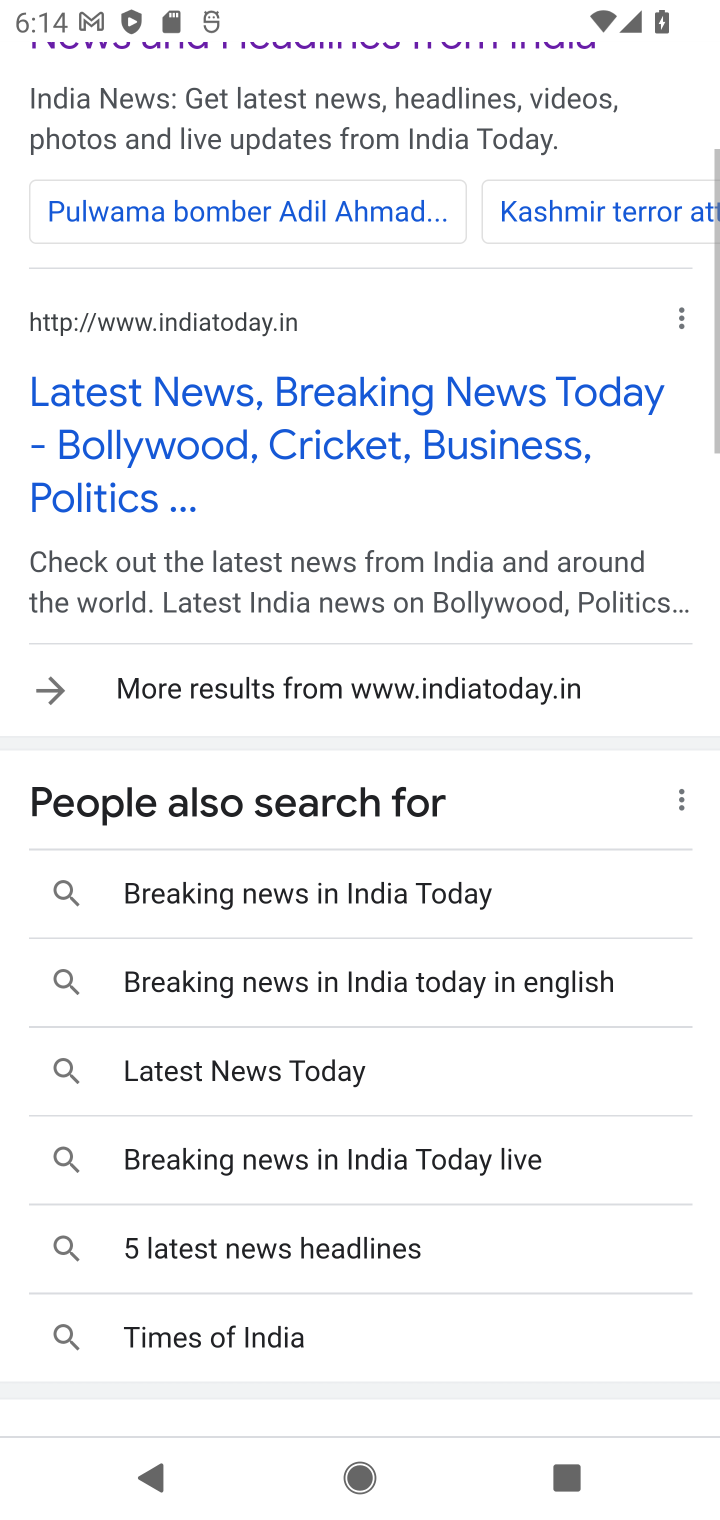
Step 26: click (586, 570)
Your task to perform on an android device: What's the news in India? Image 27: 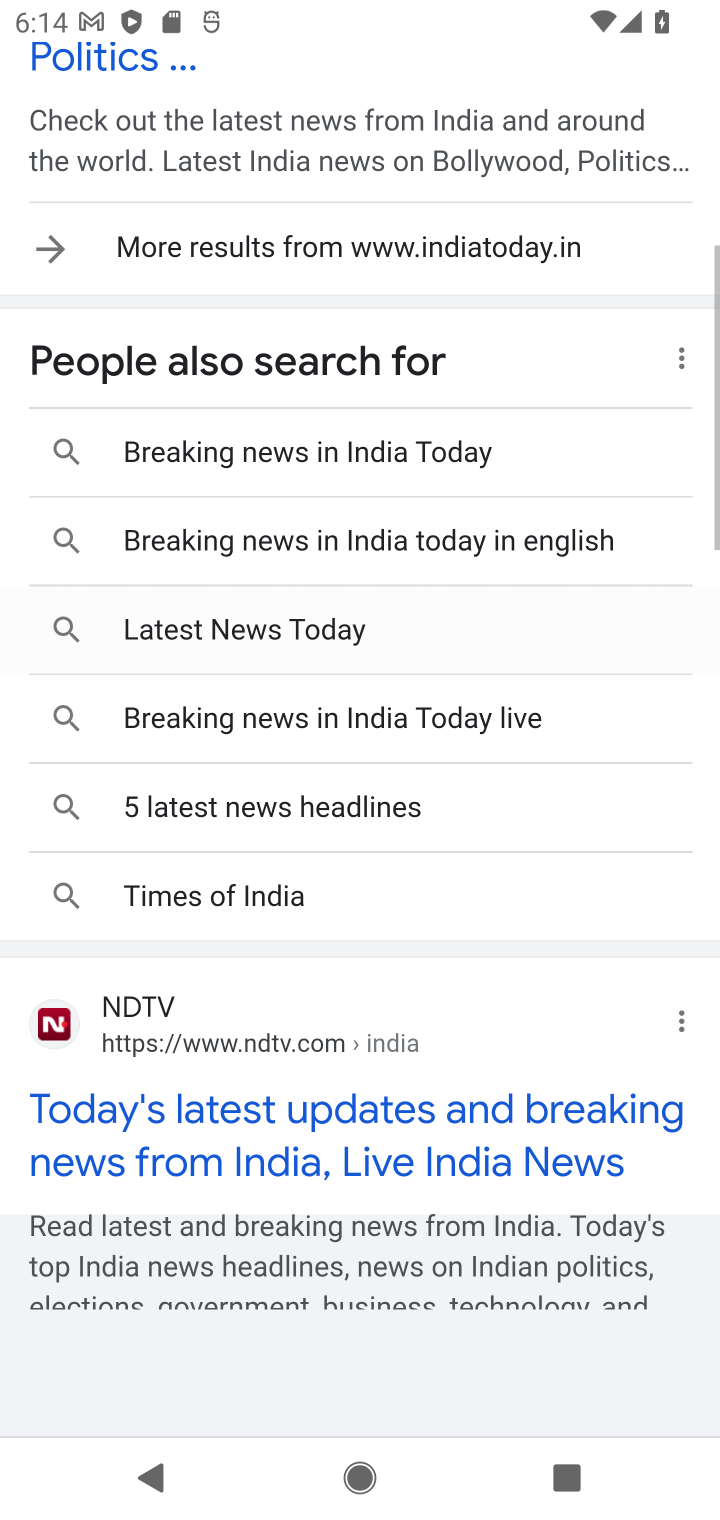
Step 27: drag from (560, 764) to (581, 643)
Your task to perform on an android device: What's the news in India? Image 28: 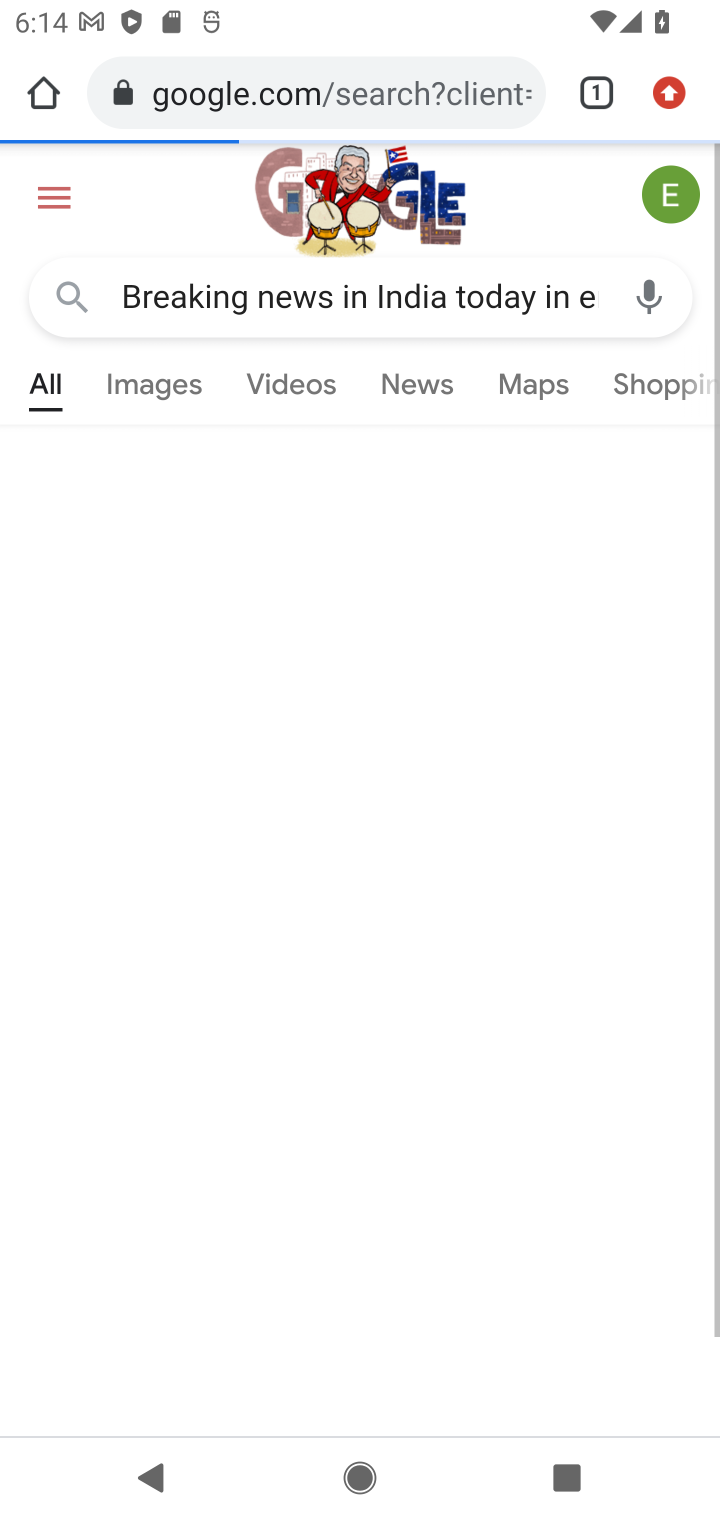
Step 28: drag from (617, 765) to (617, 657)
Your task to perform on an android device: What's the news in India? Image 29: 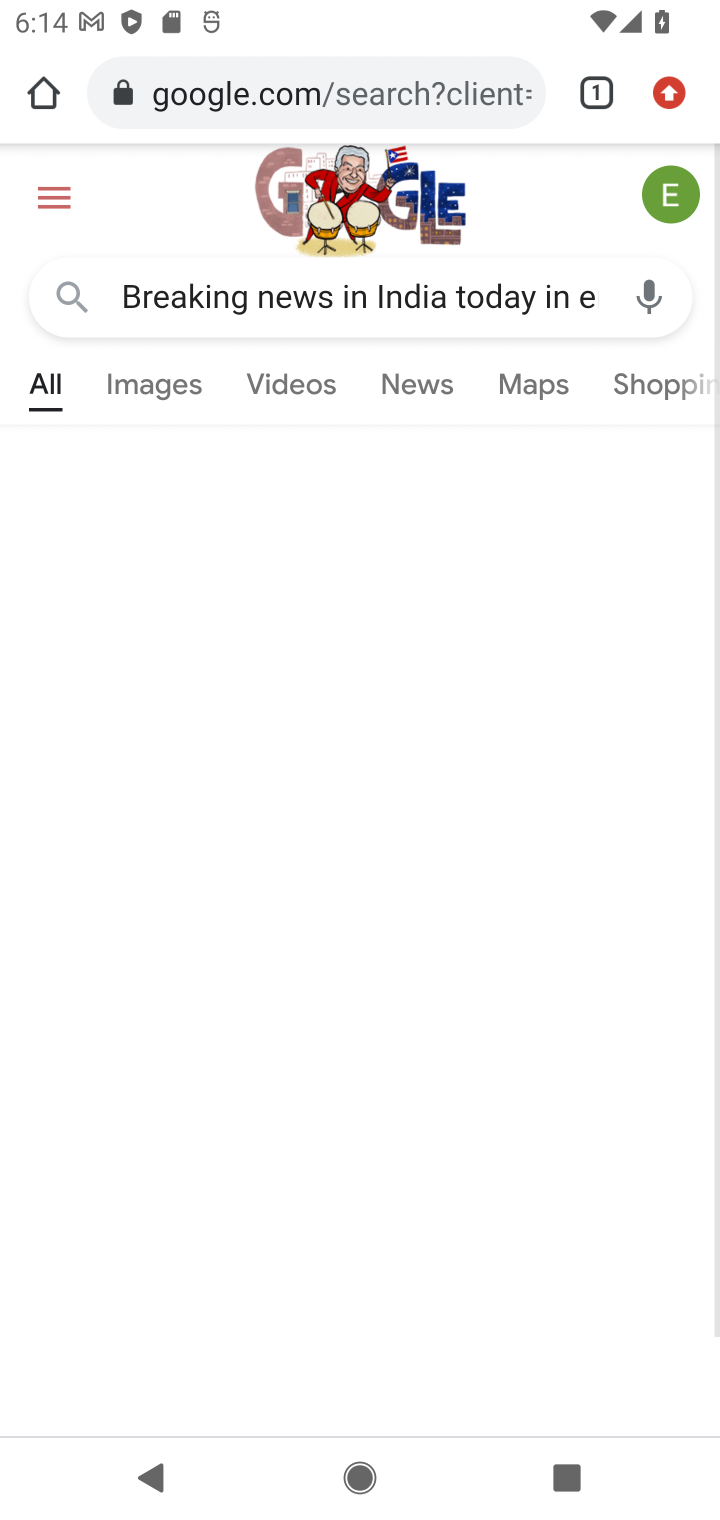
Step 29: drag from (600, 831) to (622, 647)
Your task to perform on an android device: What's the news in India? Image 30: 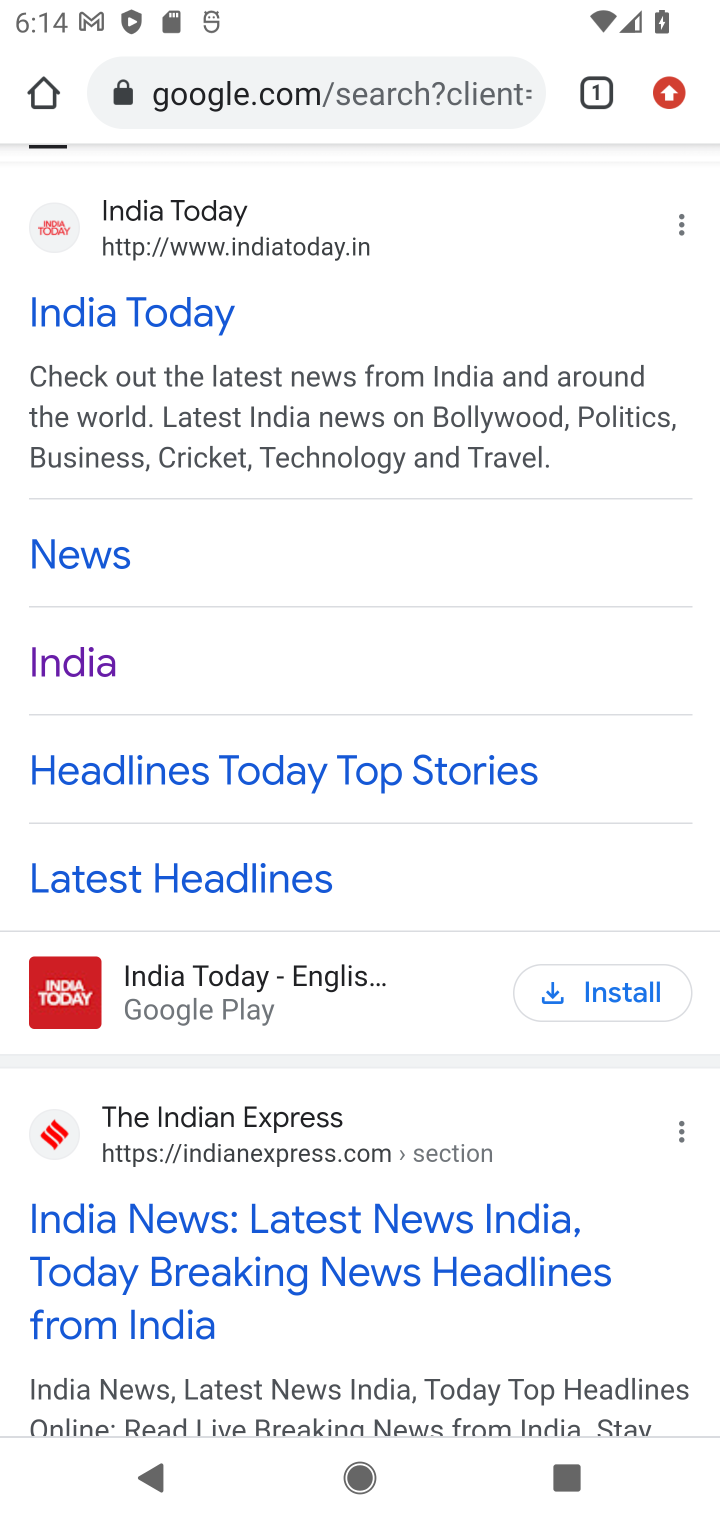
Step 30: drag from (638, 935) to (673, 627)
Your task to perform on an android device: What's the news in India? Image 31: 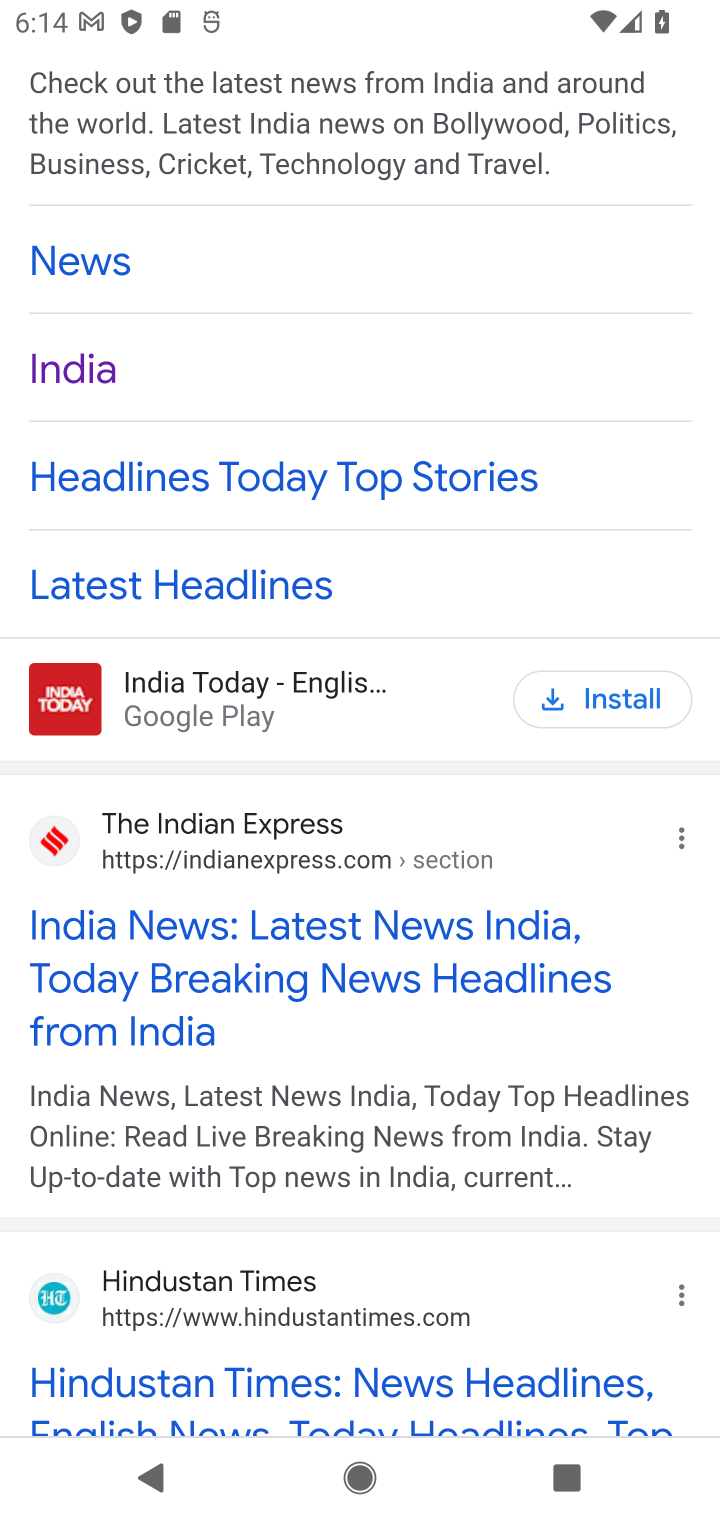
Step 31: drag from (562, 1183) to (585, 670)
Your task to perform on an android device: What's the news in India? Image 32: 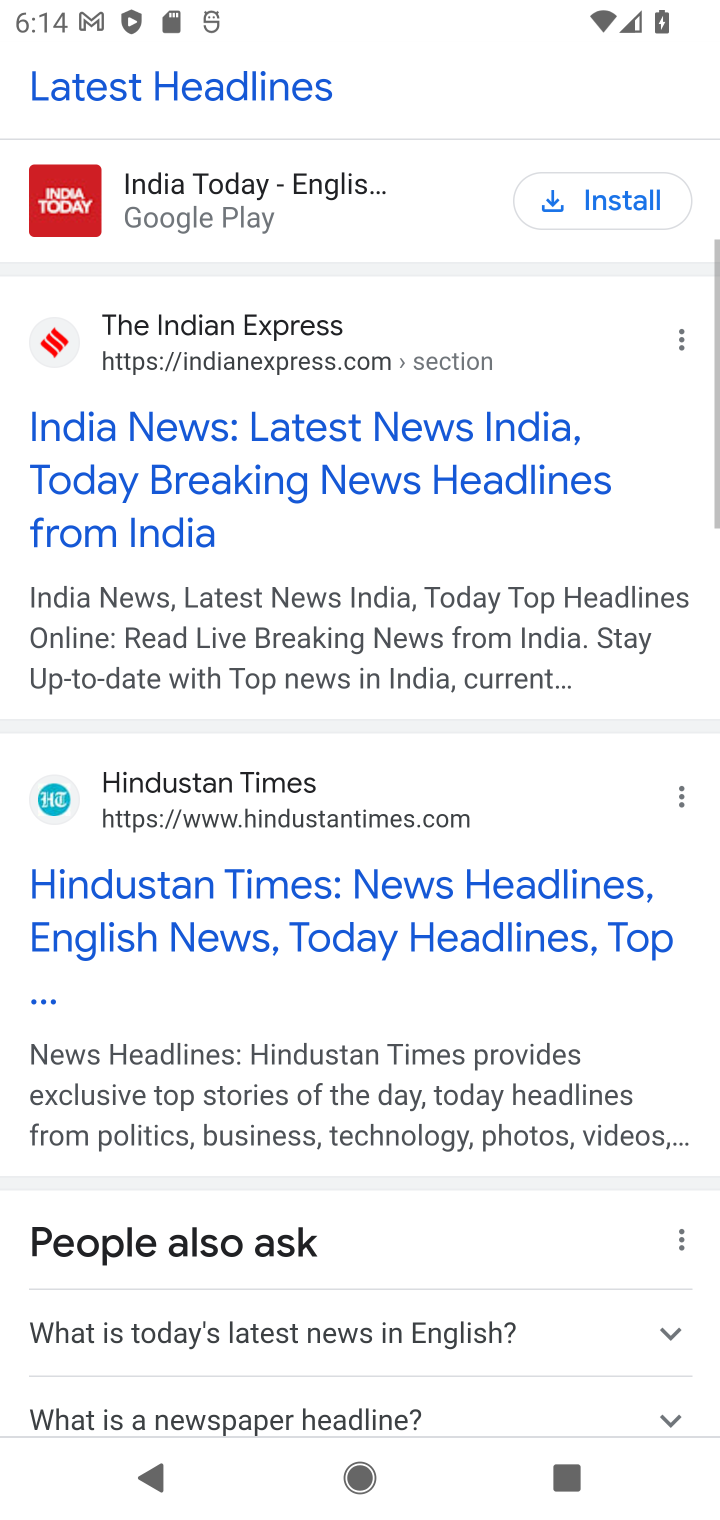
Step 32: drag from (543, 1282) to (547, 750)
Your task to perform on an android device: What's the news in India? Image 33: 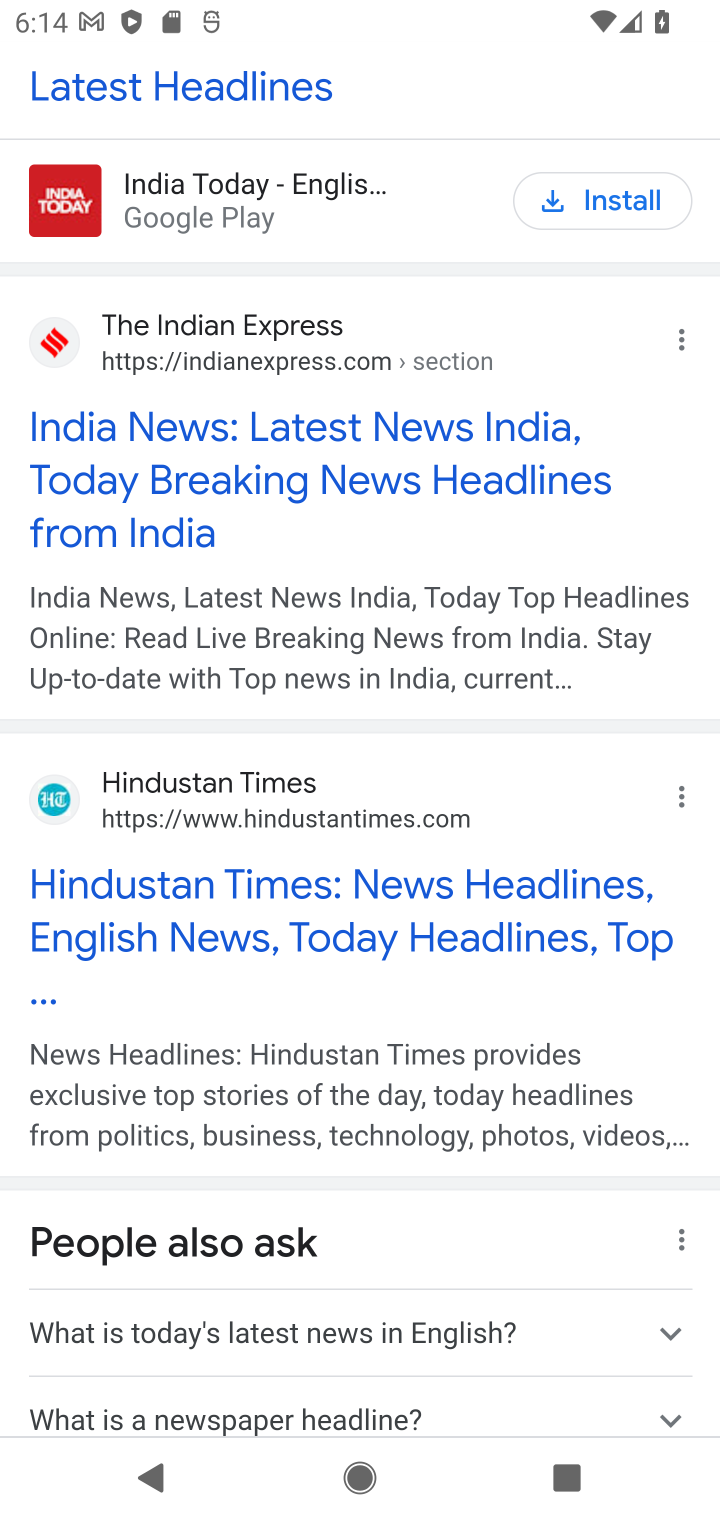
Step 33: drag from (509, 1180) to (594, 506)
Your task to perform on an android device: What's the news in India? Image 34: 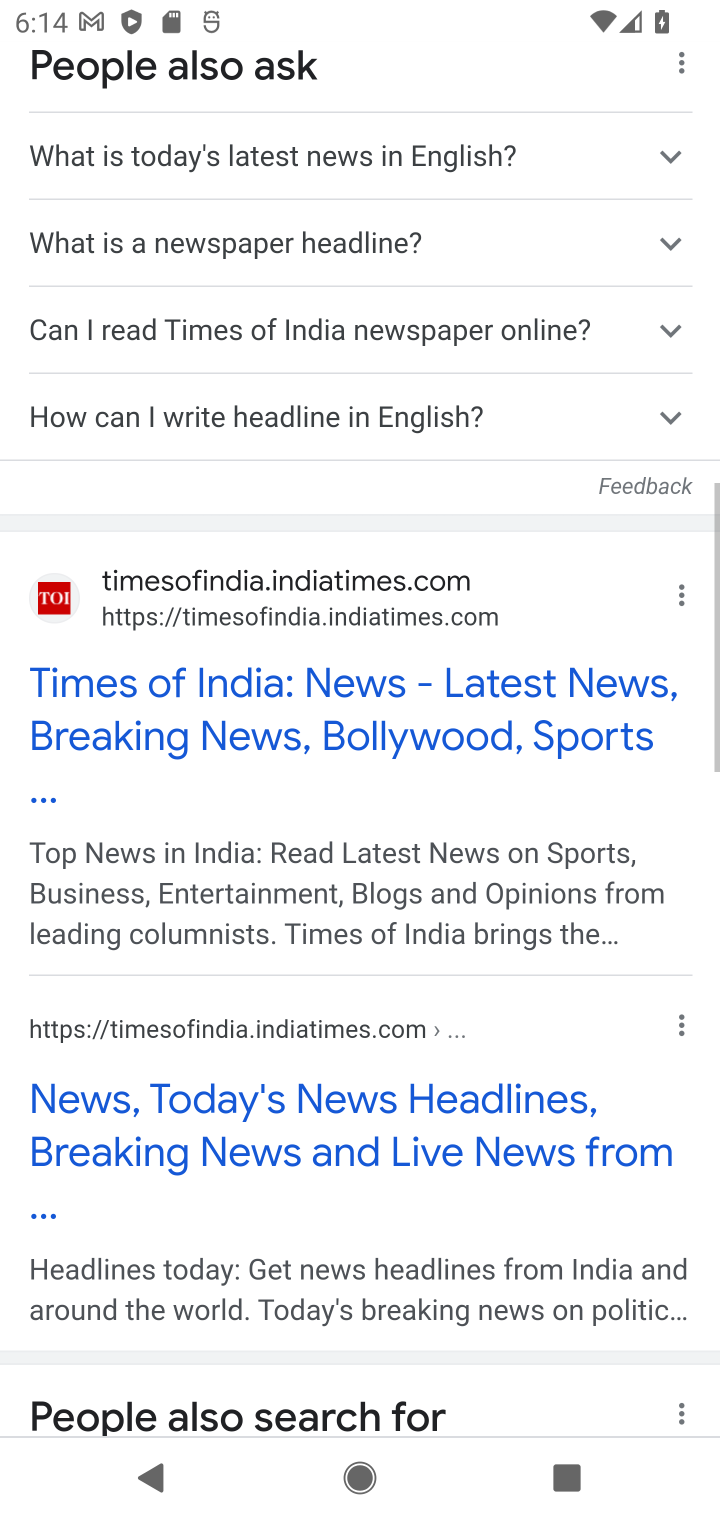
Step 34: drag from (487, 1199) to (496, 679)
Your task to perform on an android device: What's the news in India? Image 35: 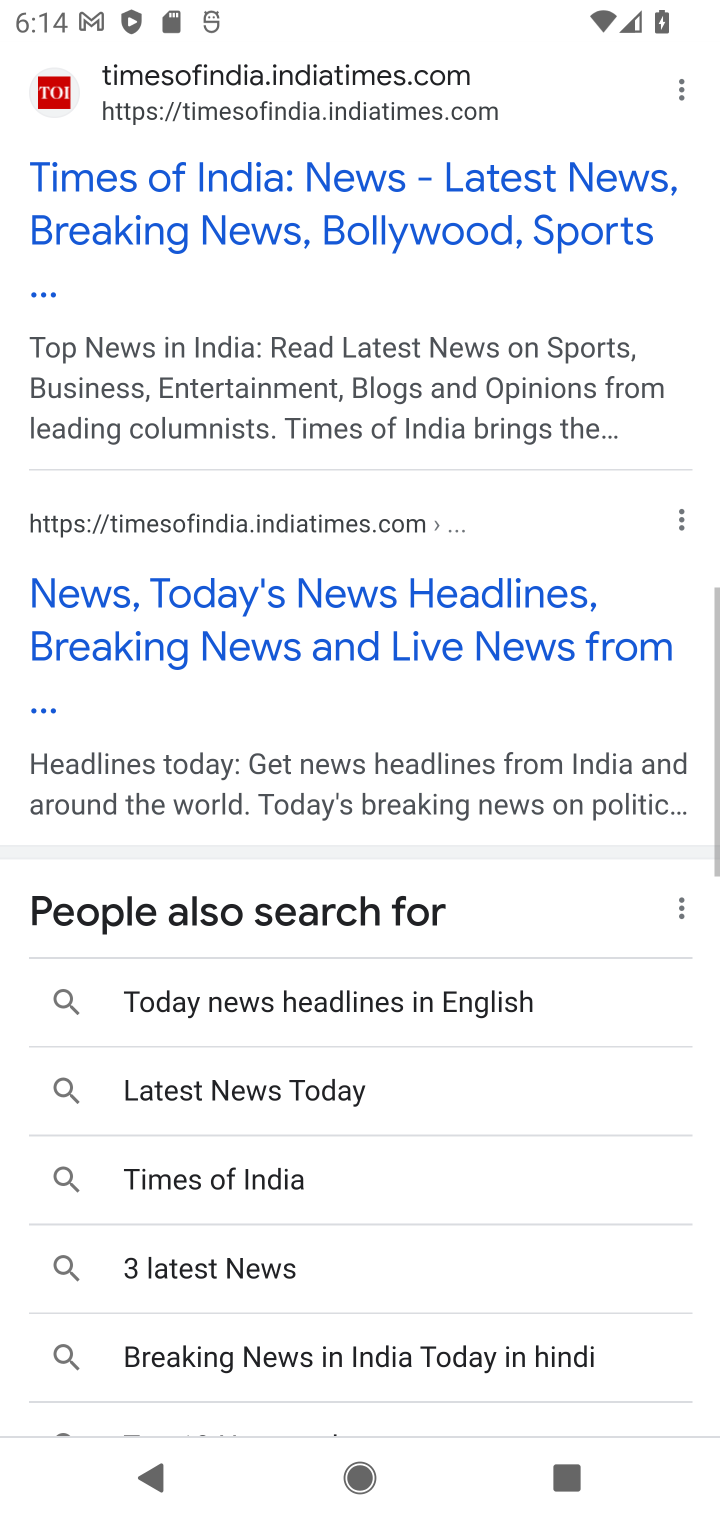
Step 35: drag from (570, 1058) to (594, 645)
Your task to perform on an android device: What's the news in India? Image 36: 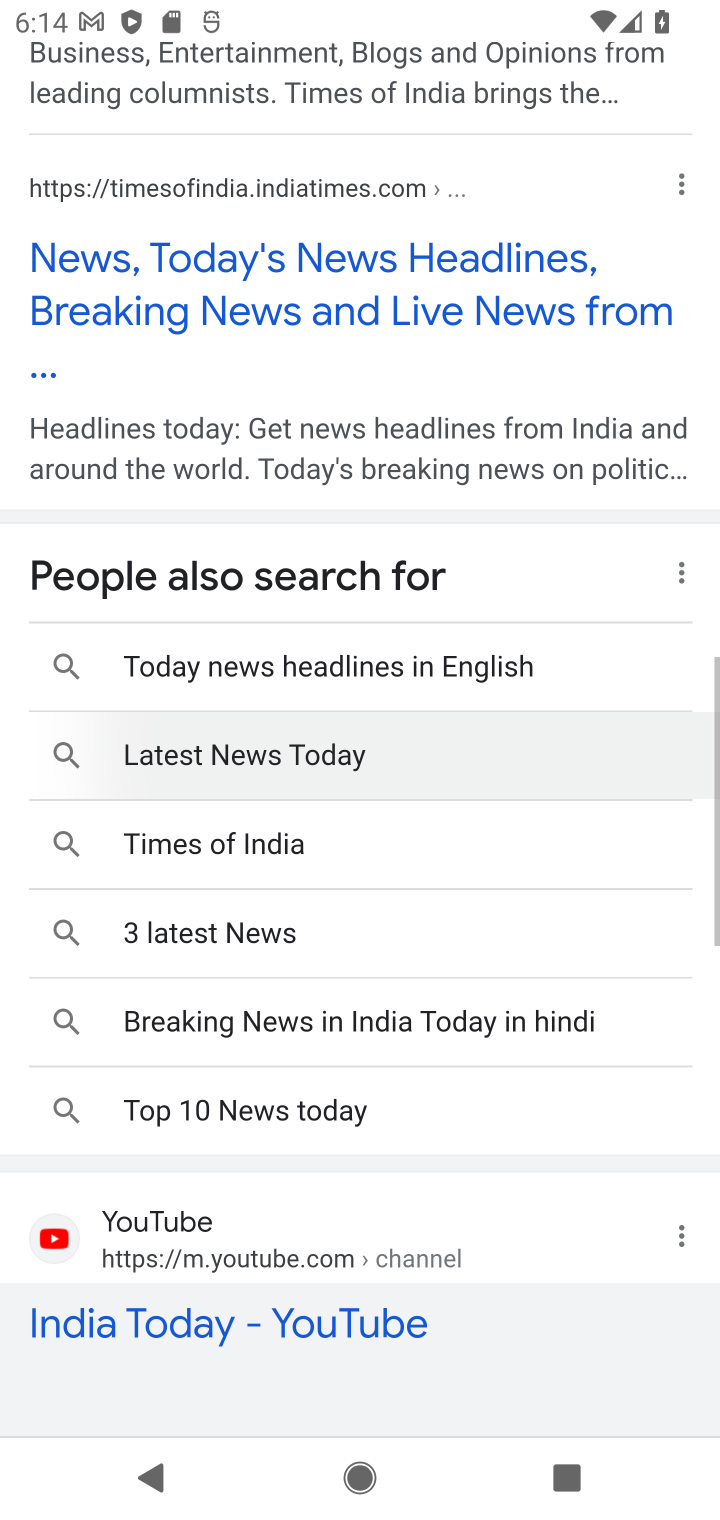
Step 36: drag from (650, 1120) to (682, 507)
Your task to perform on an android device: What's the news in India? Image 37: 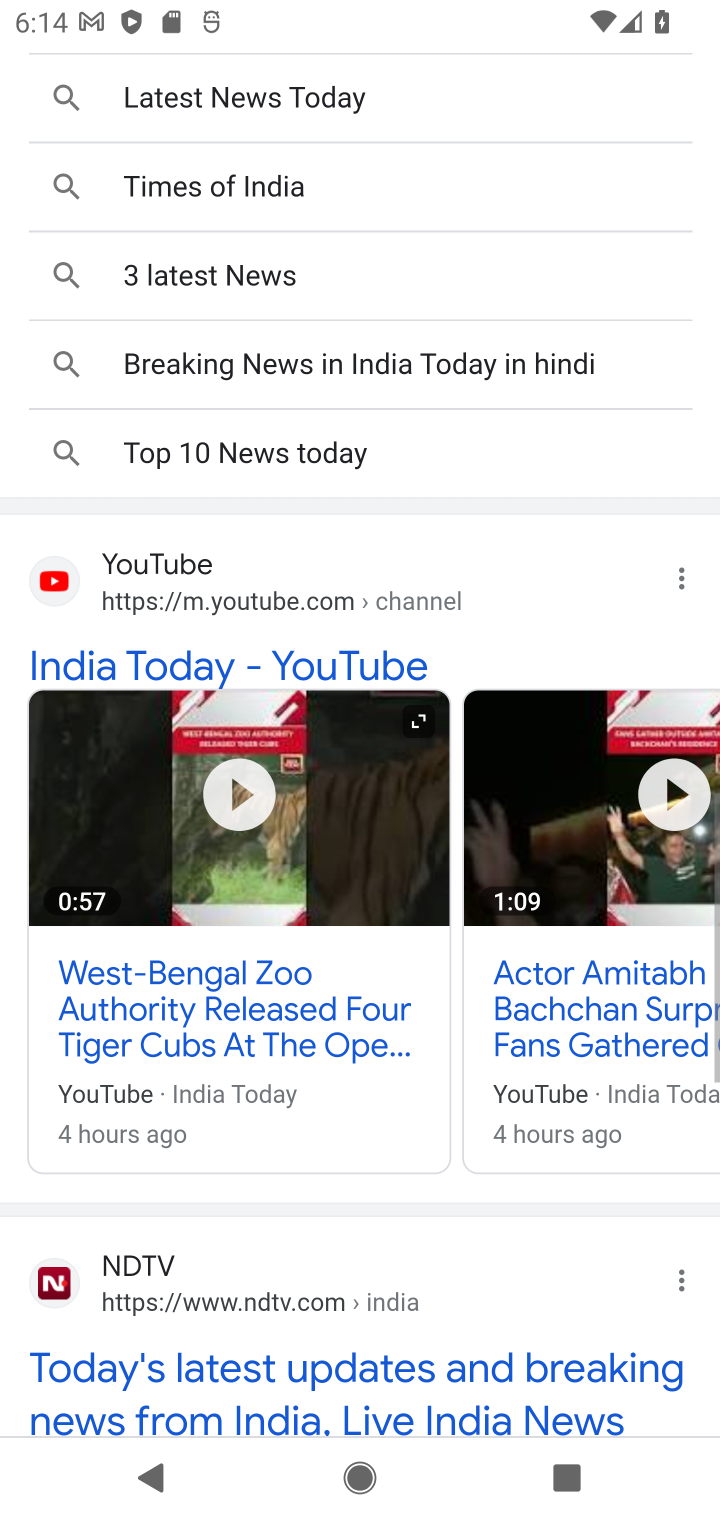
Step 37: drag from (627, 980) to (574, 656)
Your task to perform on an android device: What's the news in India? Image 38: 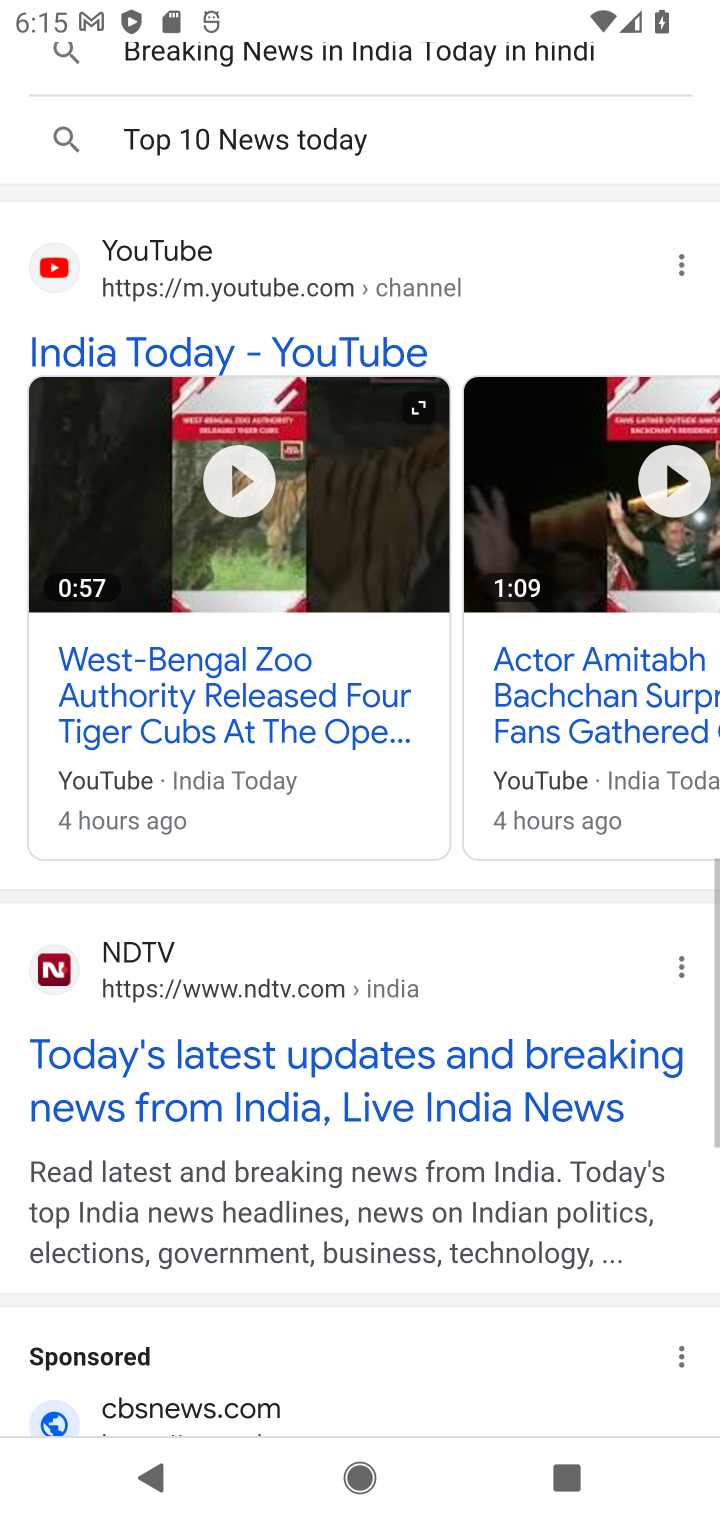
Step 38: click (484, 1026)
Your task to perform on an android device: What's the news in India? Image 39: 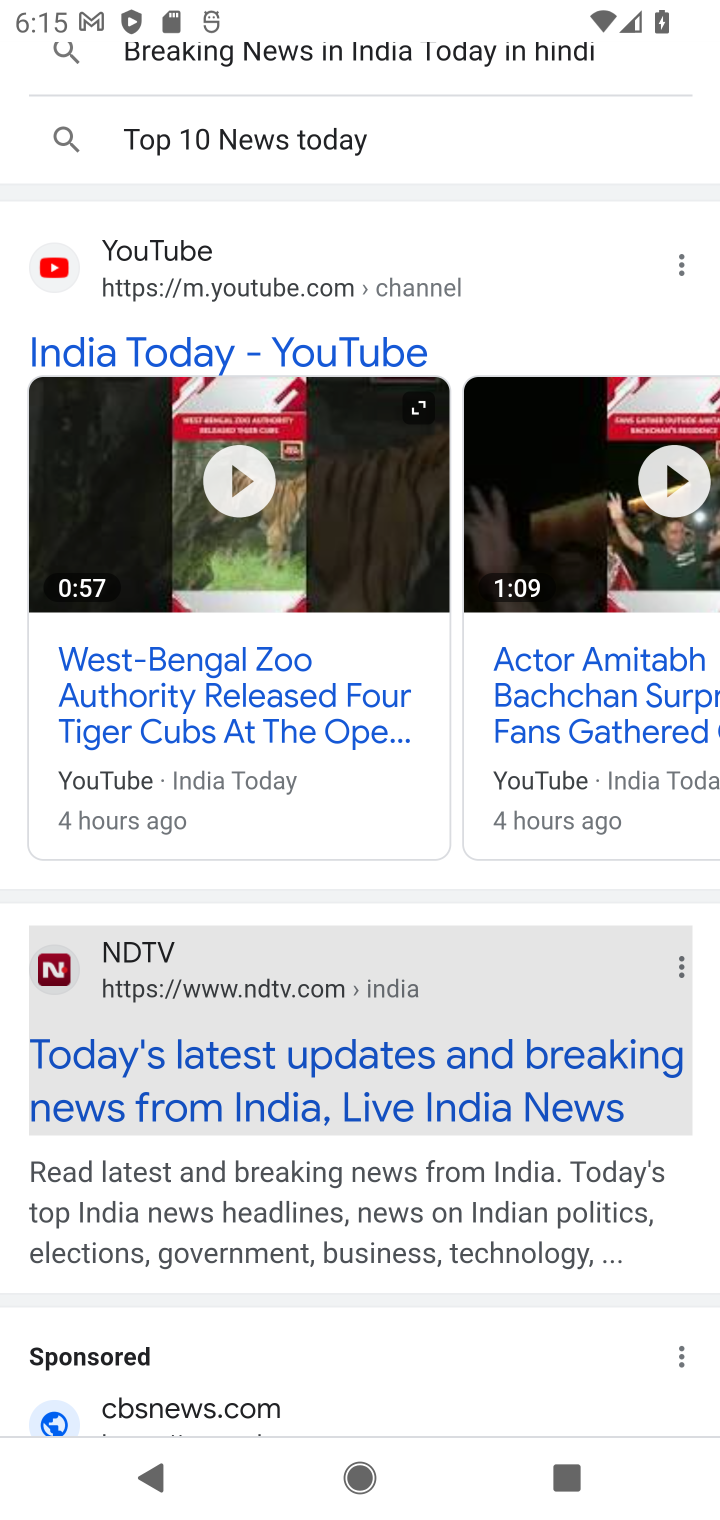
Step 39: click (341, 1028)
Your task to perform on an android device: What's the news in India? Image 40: 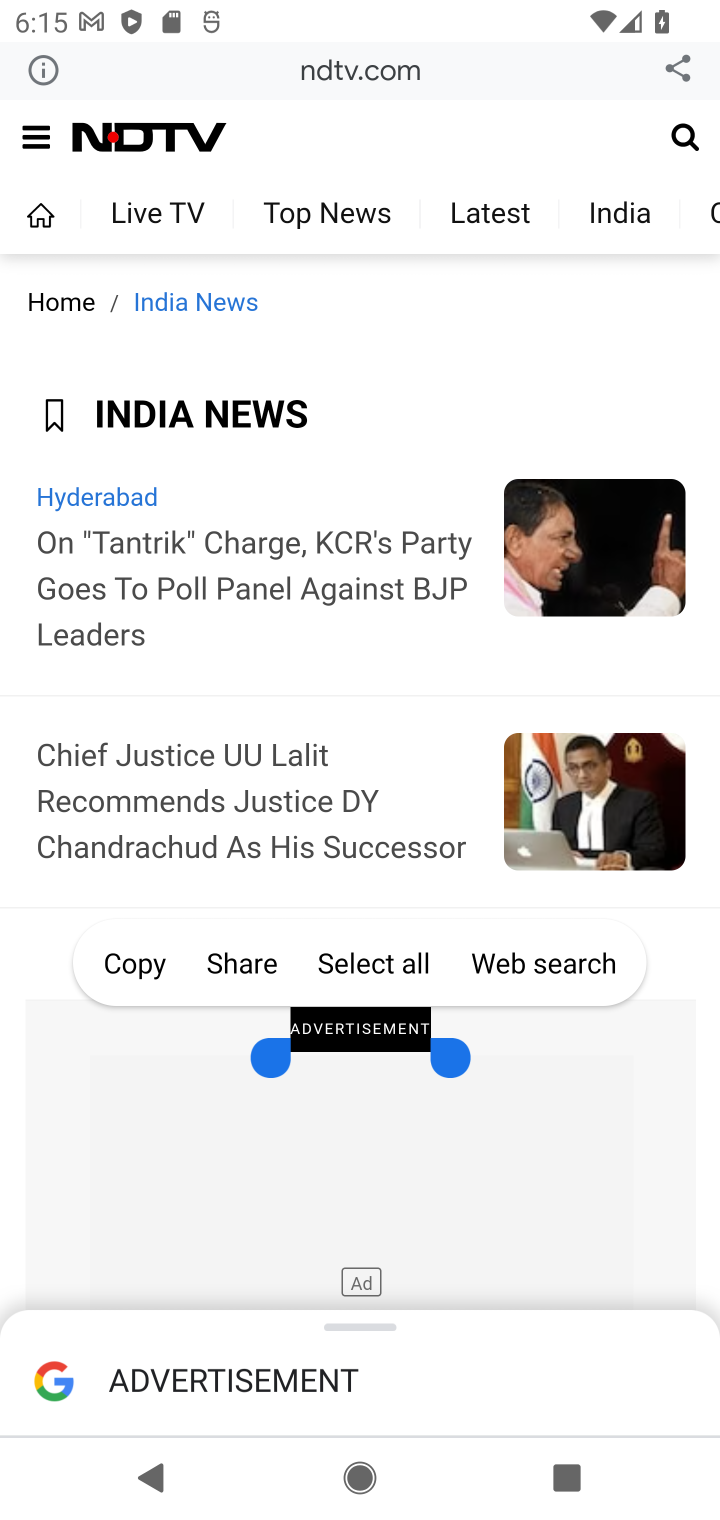
Step 40: click (477, 1274)
Your task to perform on an android device: What's the news in India? Image 41: 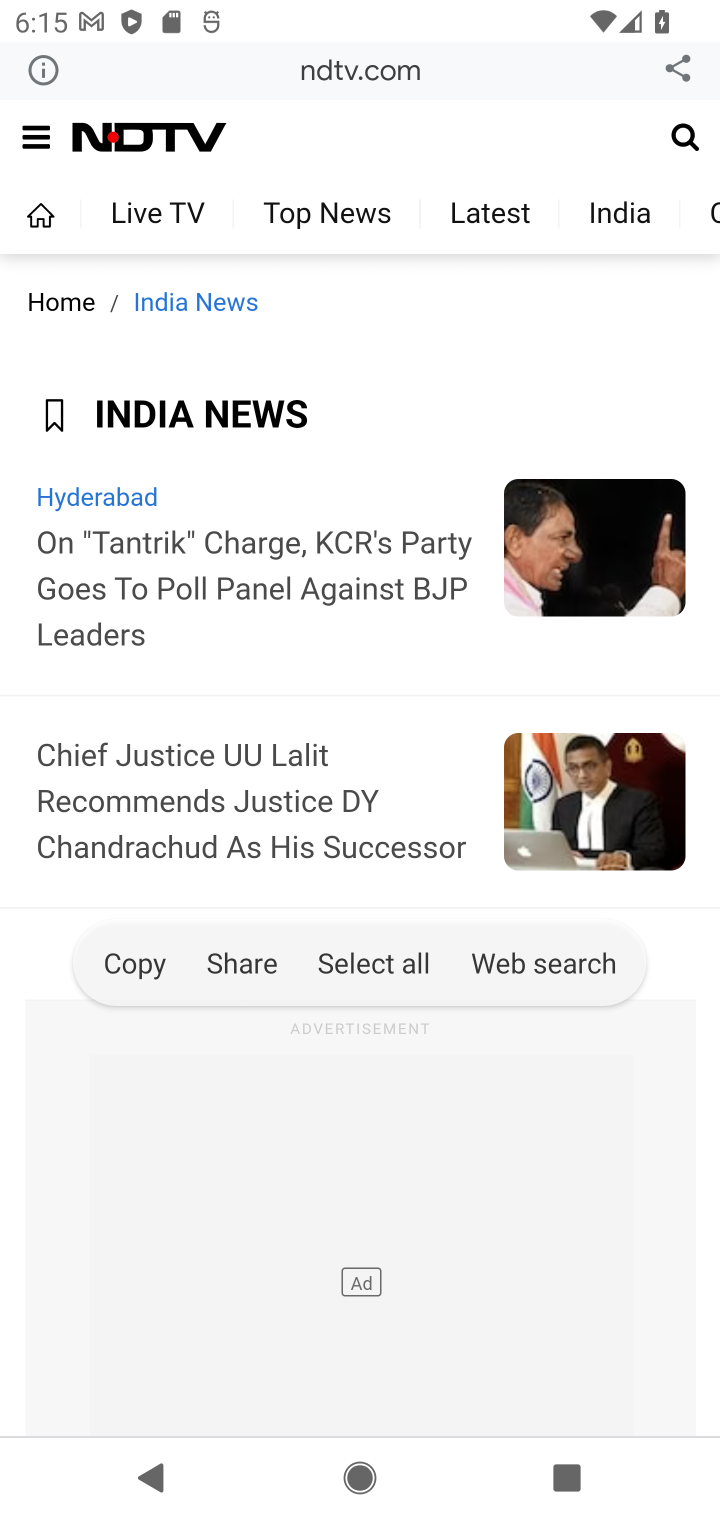
Step 41: click (542, 1224)
Your task to perform on an android device: What's the news in India? Image 42: 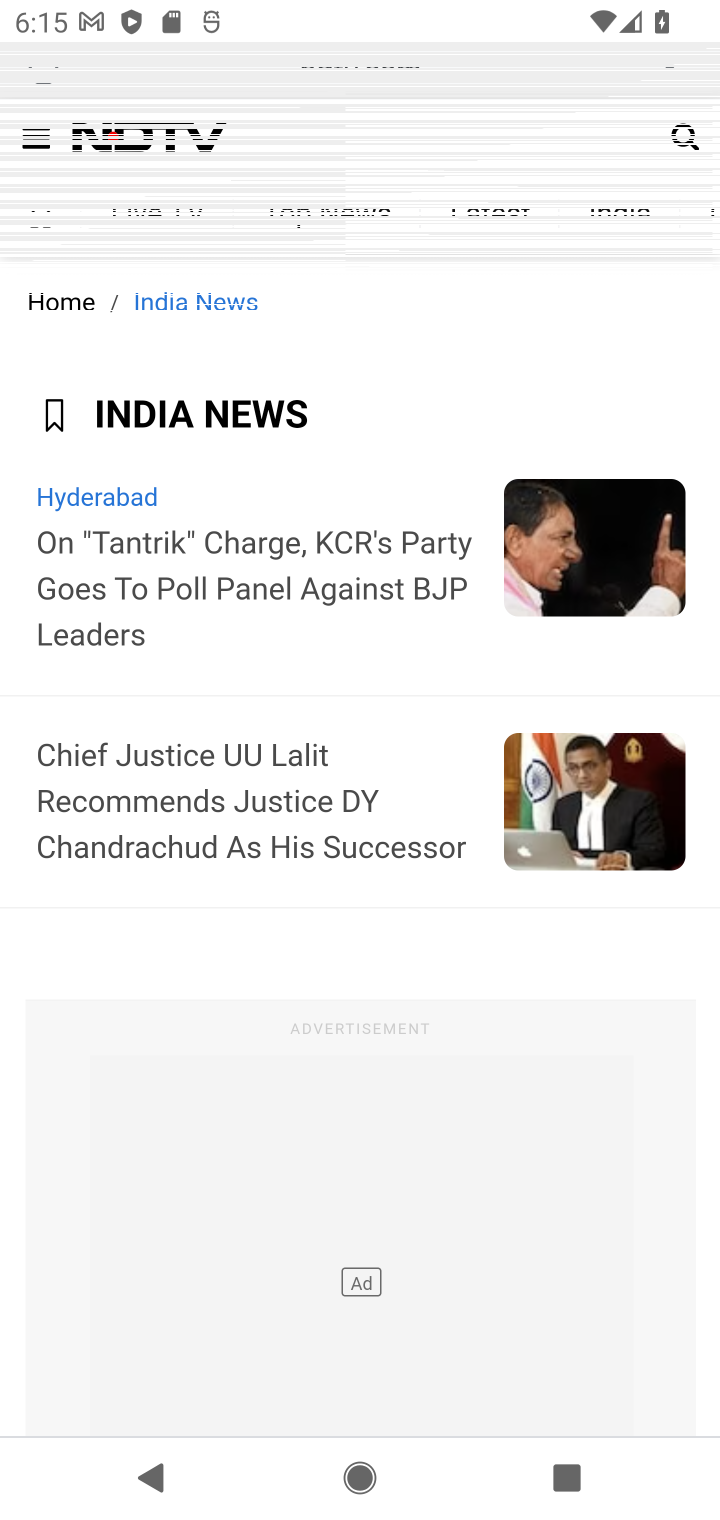
Step 42: drag from (551, 1119) to (537, 314)
Your task to perform on an android device: What's the news in India? Image 43: 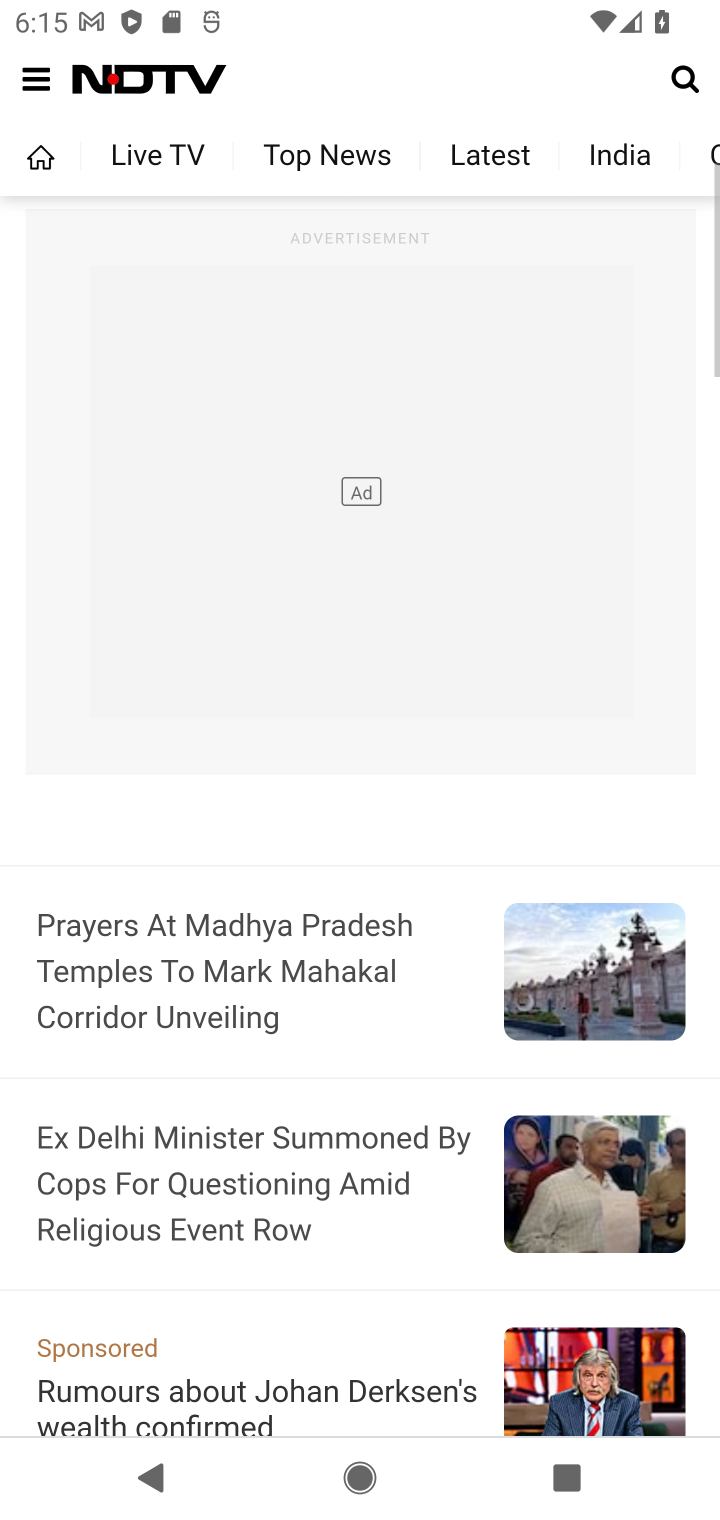
Step 43: drag from (396, 1029) to (435, 339)
Your task to perform on an android device: What's the news in India? Image 44: 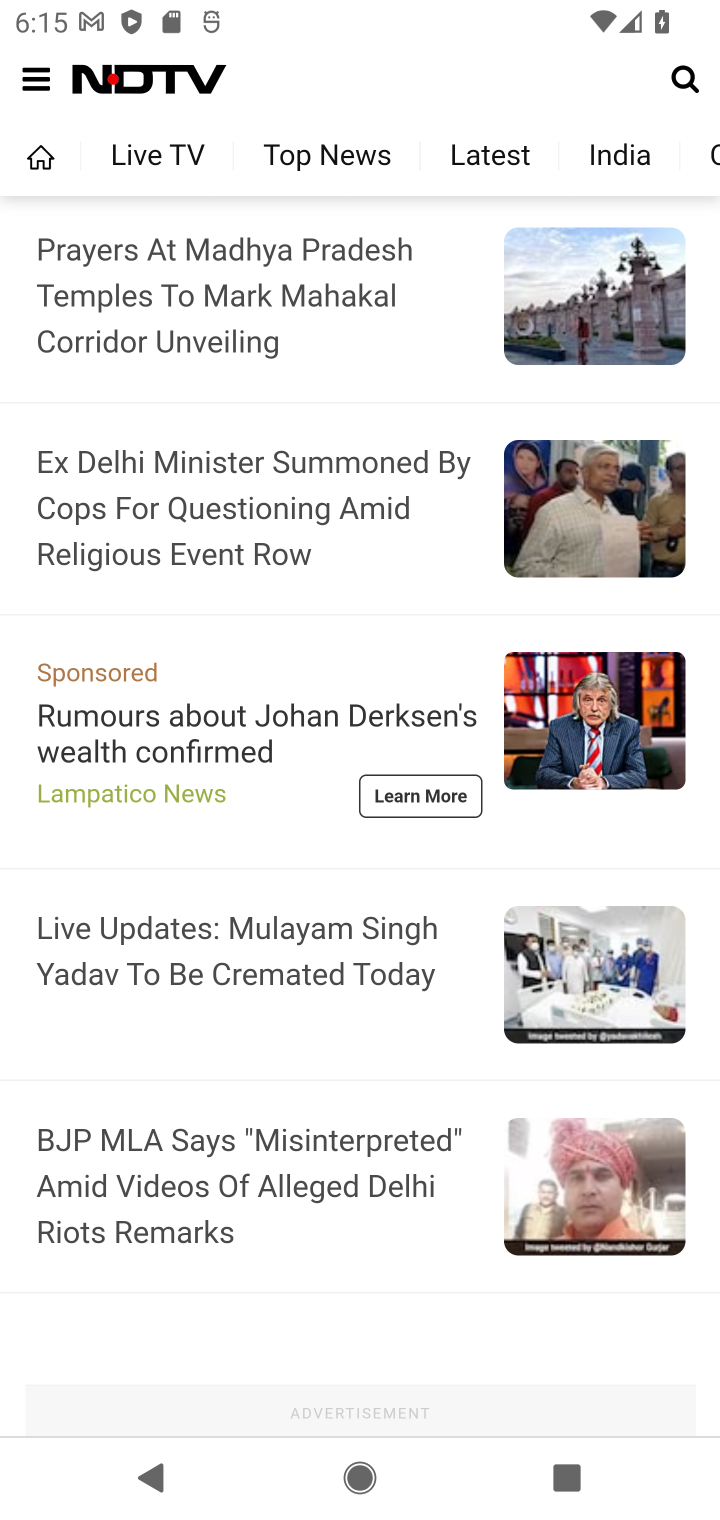
Step 44: drag from (410, 1327) to (420, 344)
Your task to perform on an android device: What's the news in India? Image 45: 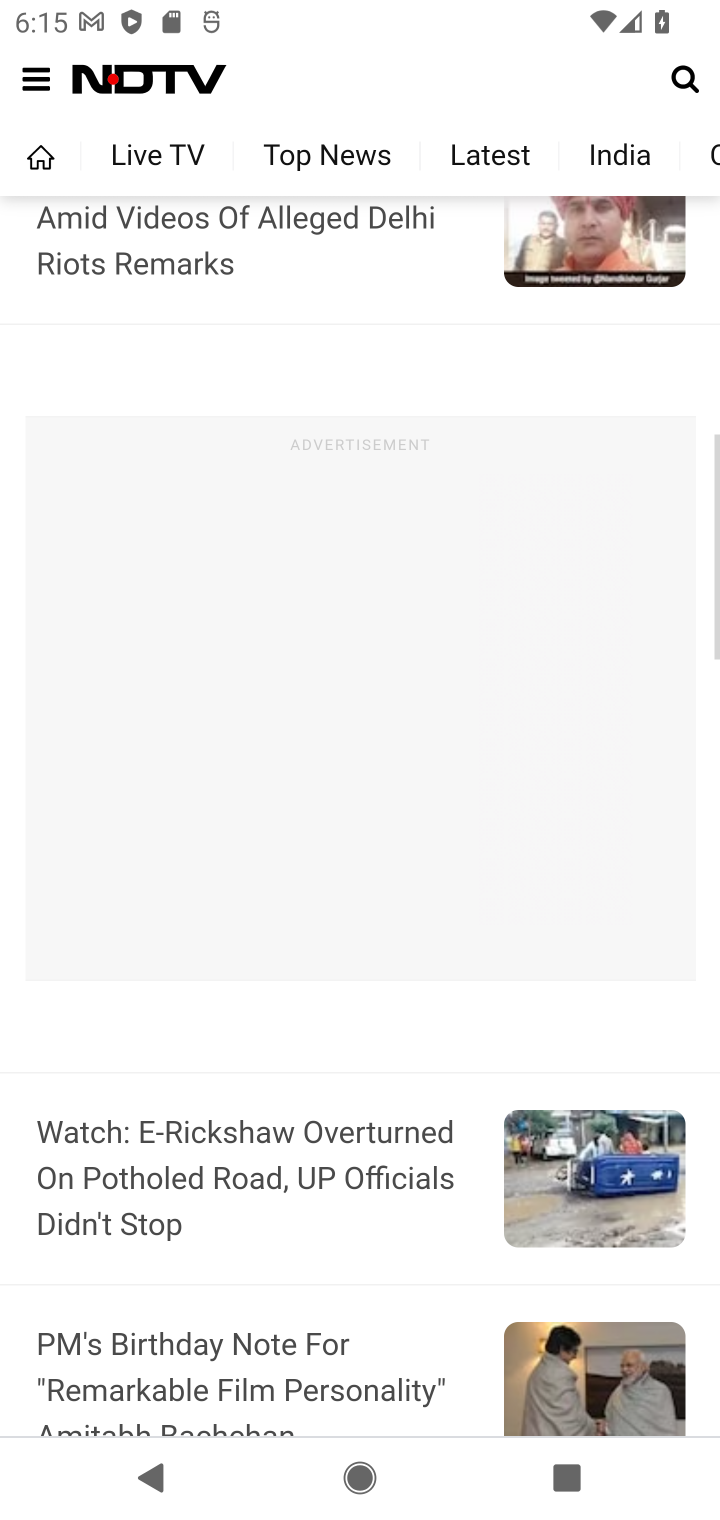
Step 45: drag from (416, 812) to (440, 289)
Your task to perform on an android device: What's the news in India? Image 46: 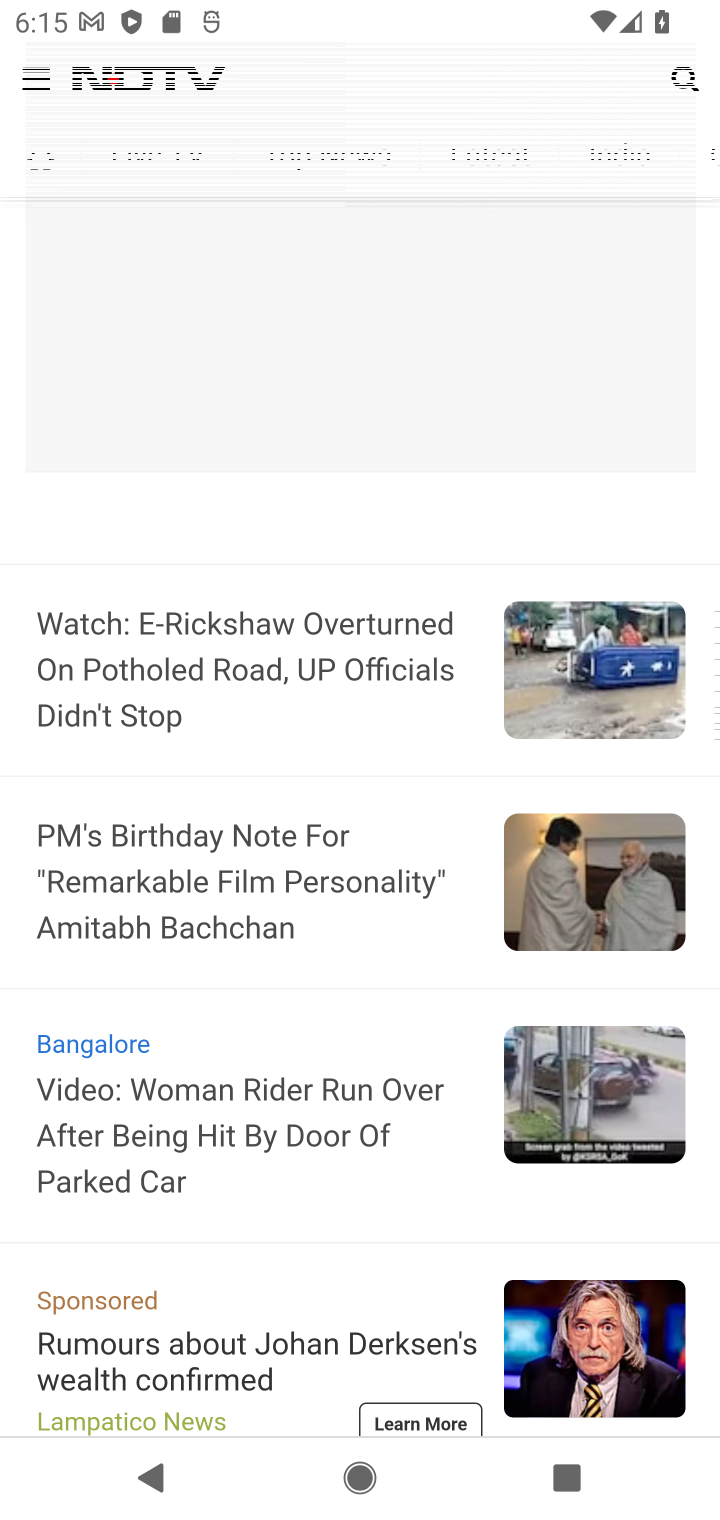
Step 46: drag from (479, 791) to (474, 344)
Your task to perform on an android device: What's the news in India? Image 47: 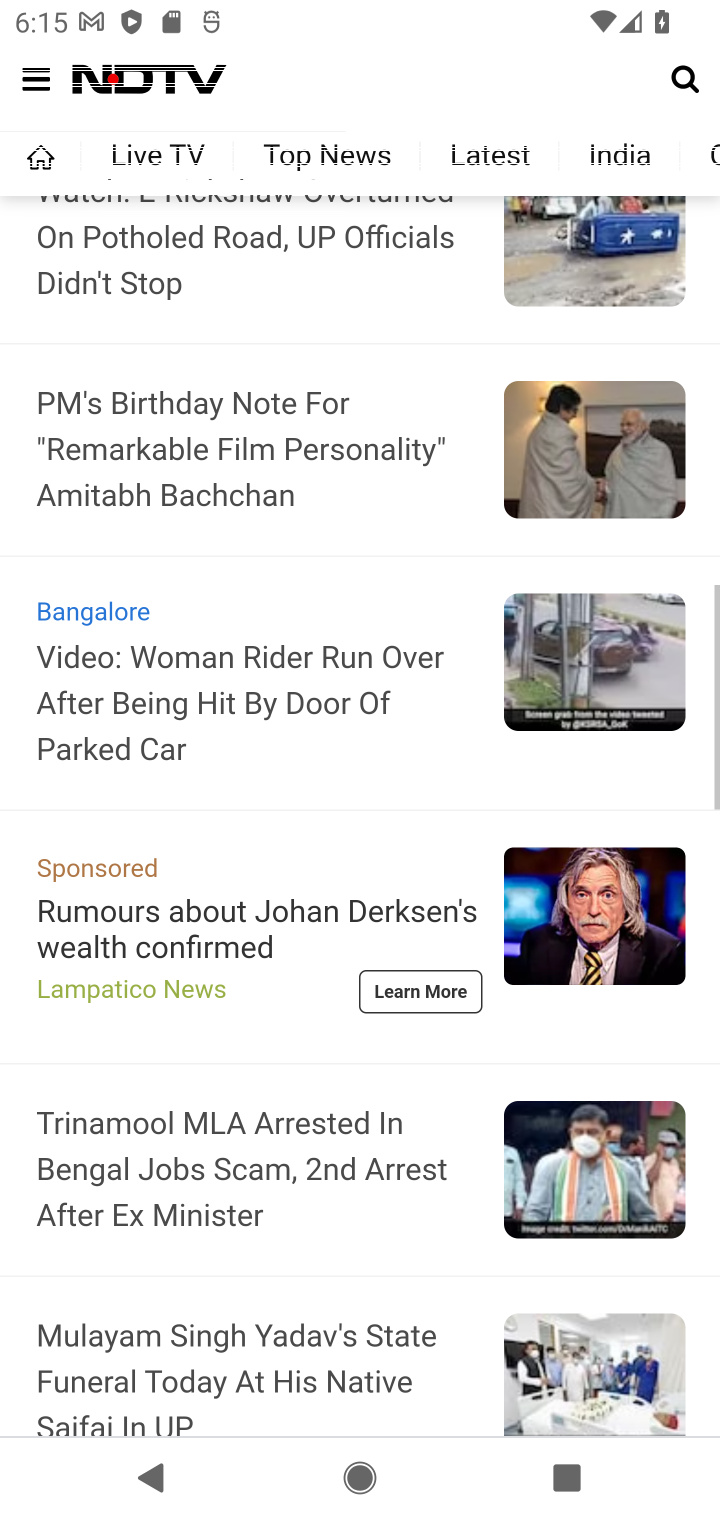
Step 47: drag from (371, 793) to (390, 438)
Your task to perform on an android device: What's the news in India? Image 48: 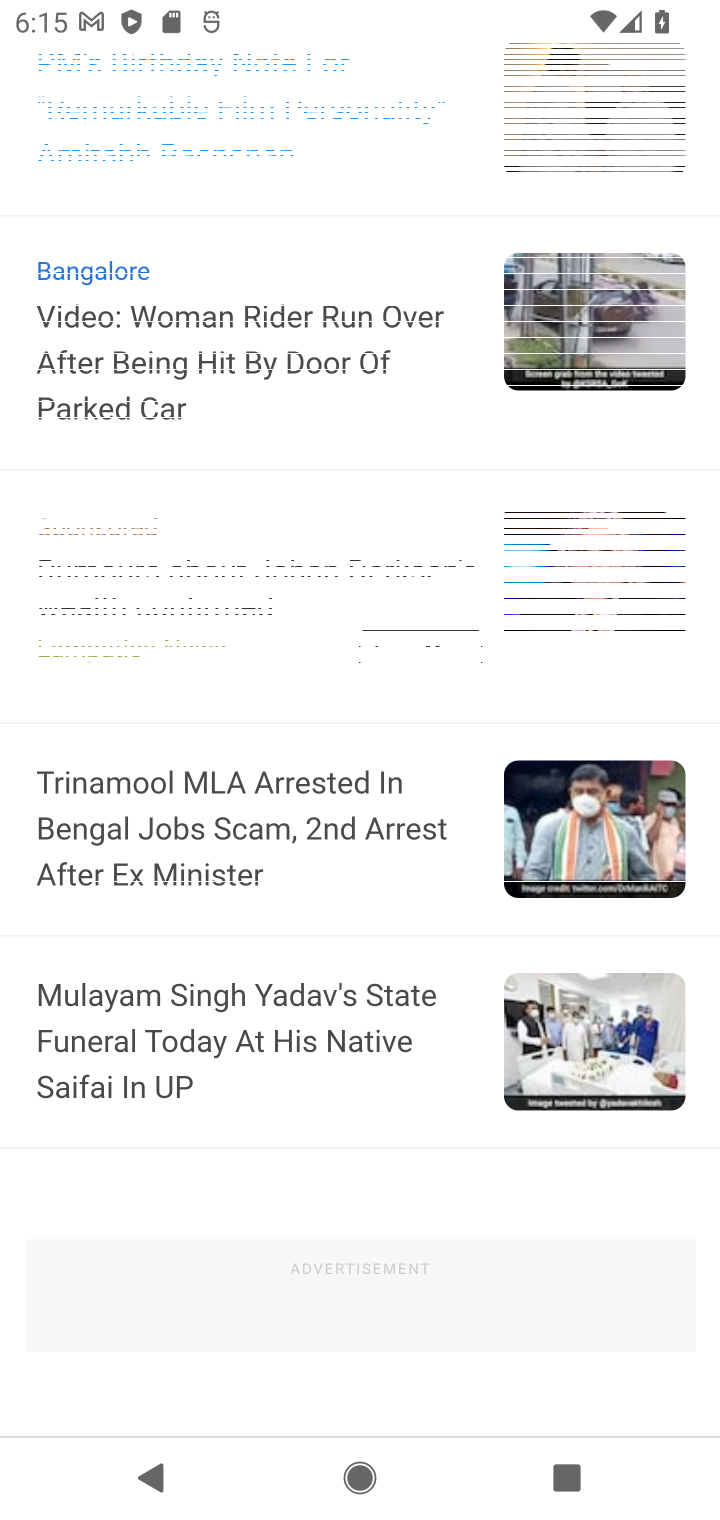
Step 48: drag from (446, 955) to (439, 415)
Your task to perform on an android device: What's the news in India? Image 49: 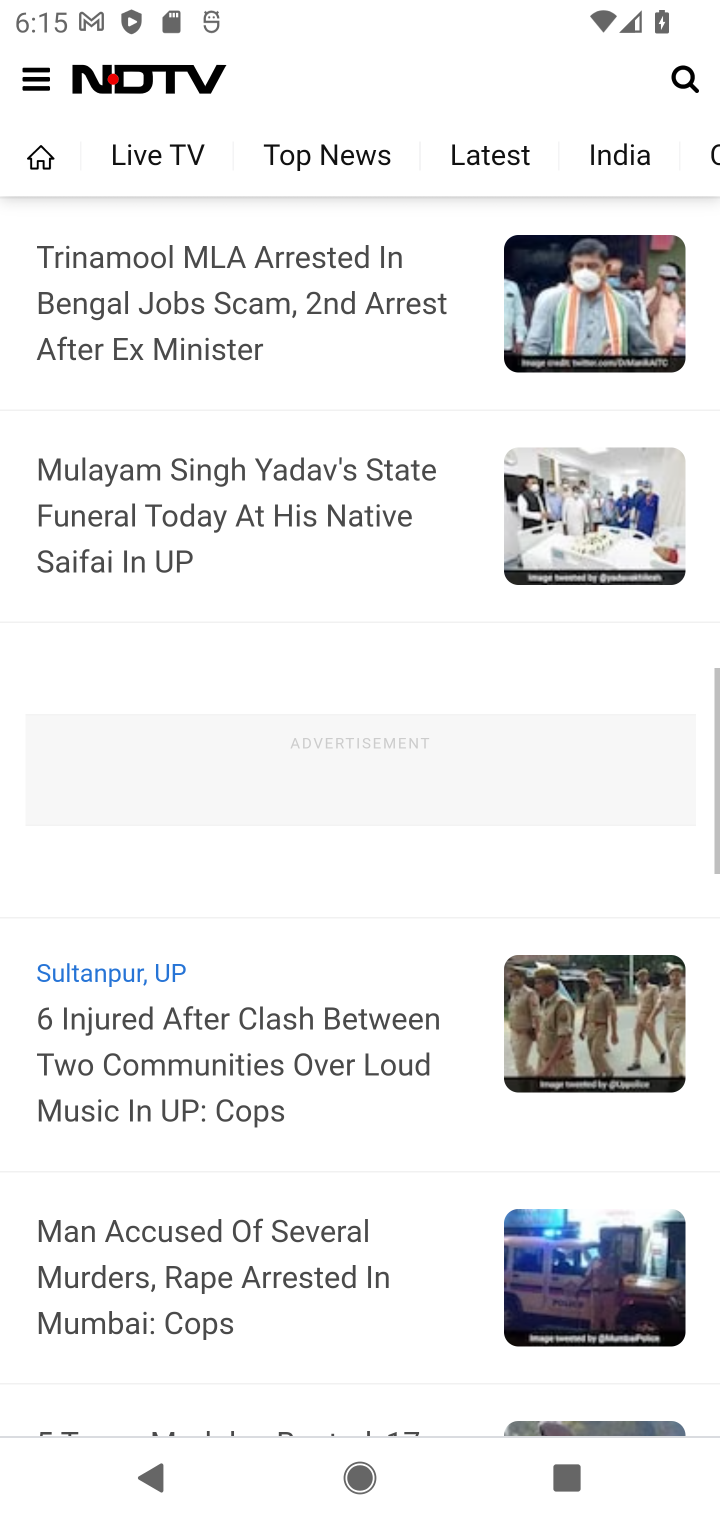
Step 49: drag from (506, 946) to (519, 571)
Your task to perform on an android device: What's the news in India? Image 50: 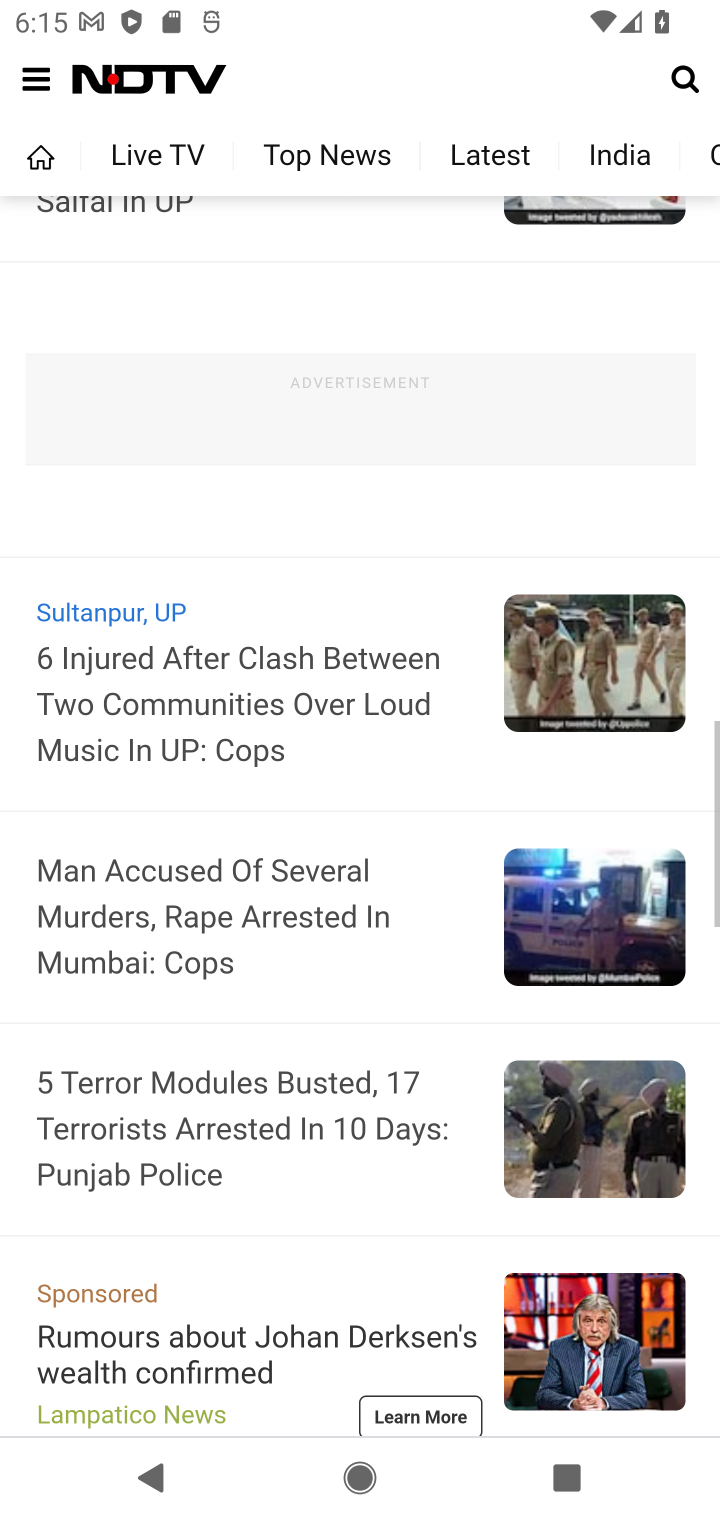
Step 50: press back button
Your task to perform on an android device: What's the news in India? Image 51: 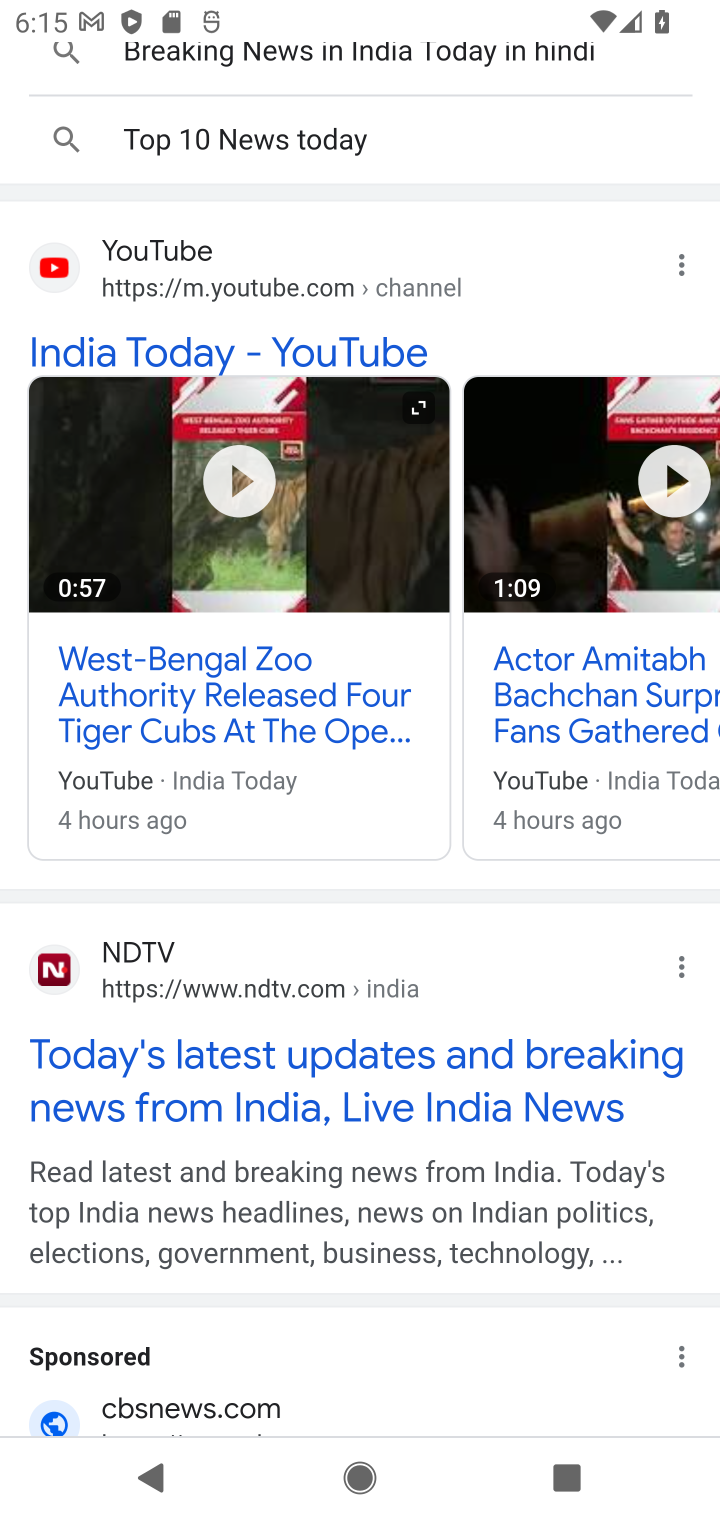
Step 51: click (478, 1086)
Your task to perform on an android device: What's the news in India? Image 52: 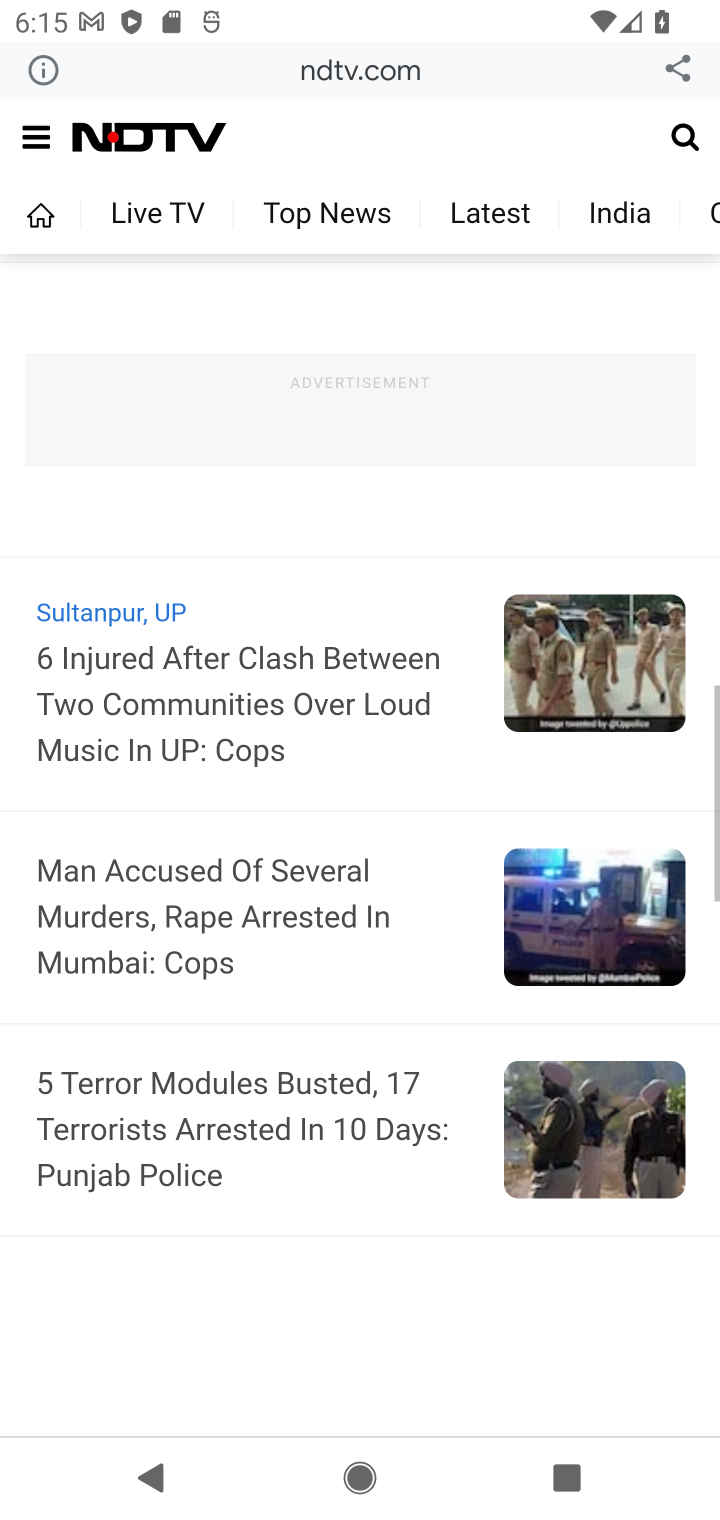
Step 52: drag from (550, 1069) to (585, 919)
Your task to perform on an android device: What's the news in India? Image 53: 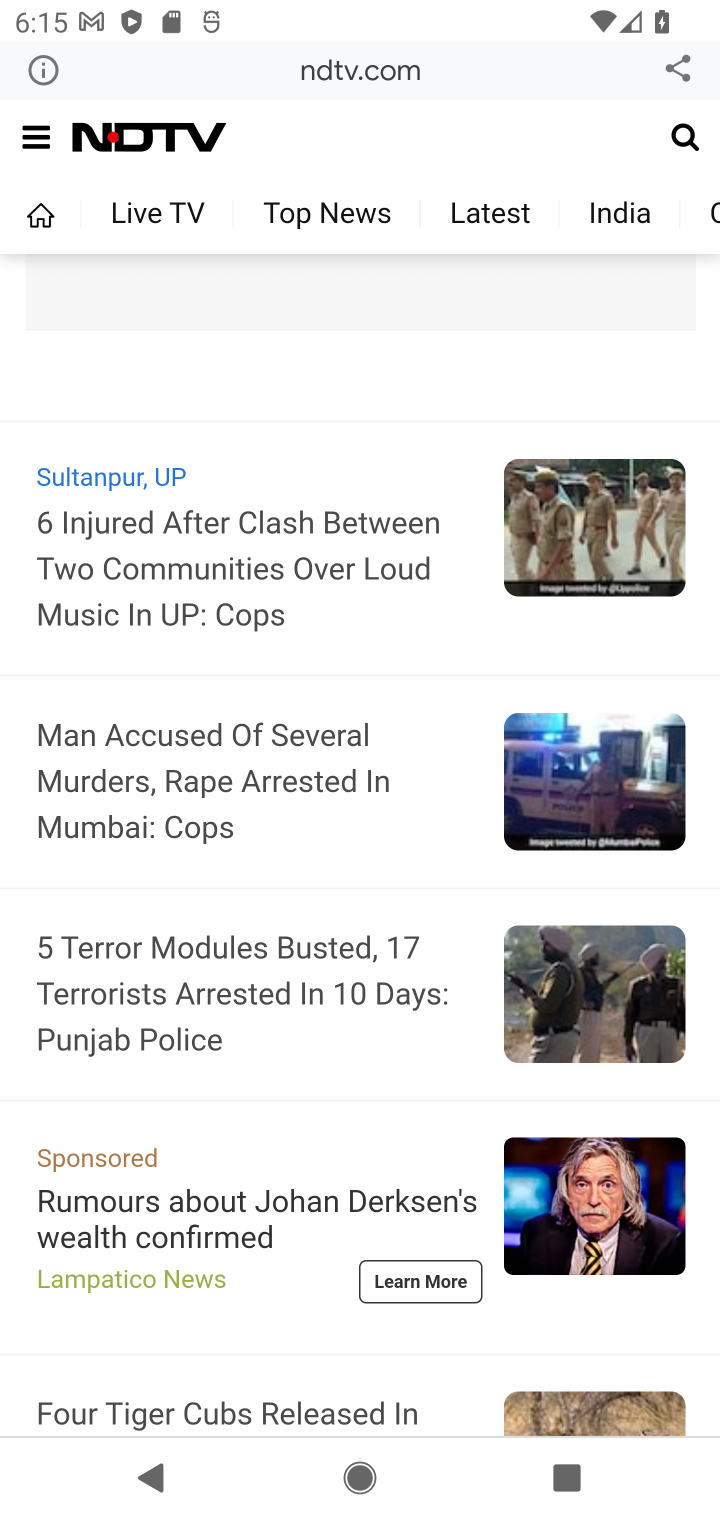
Step 53: drag from (610, 1091) to (558, 837)
Your task to perform on an android device: What's the news in India? Image 54: 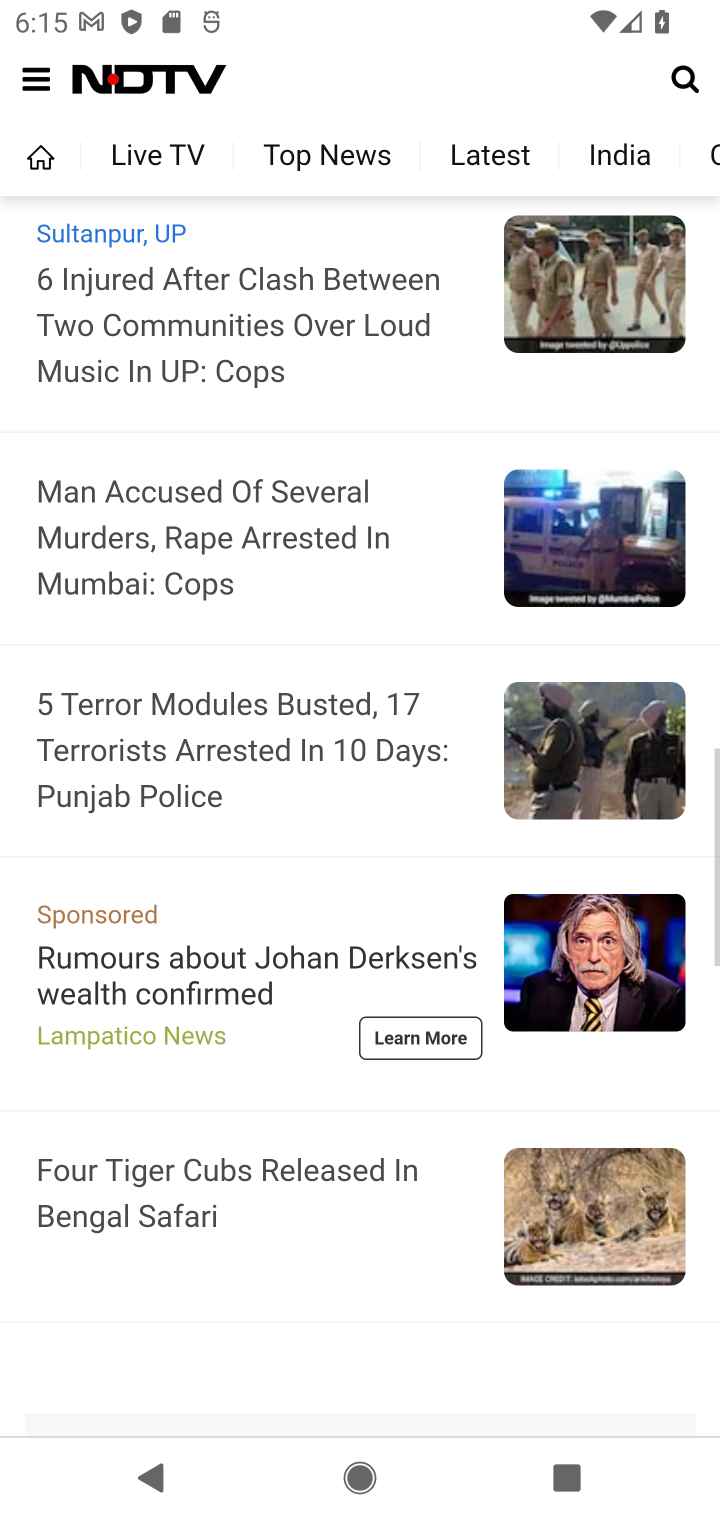
Step 54: click (592, 815)
Your task to perform on an android device: What's the news in India? Image 55: 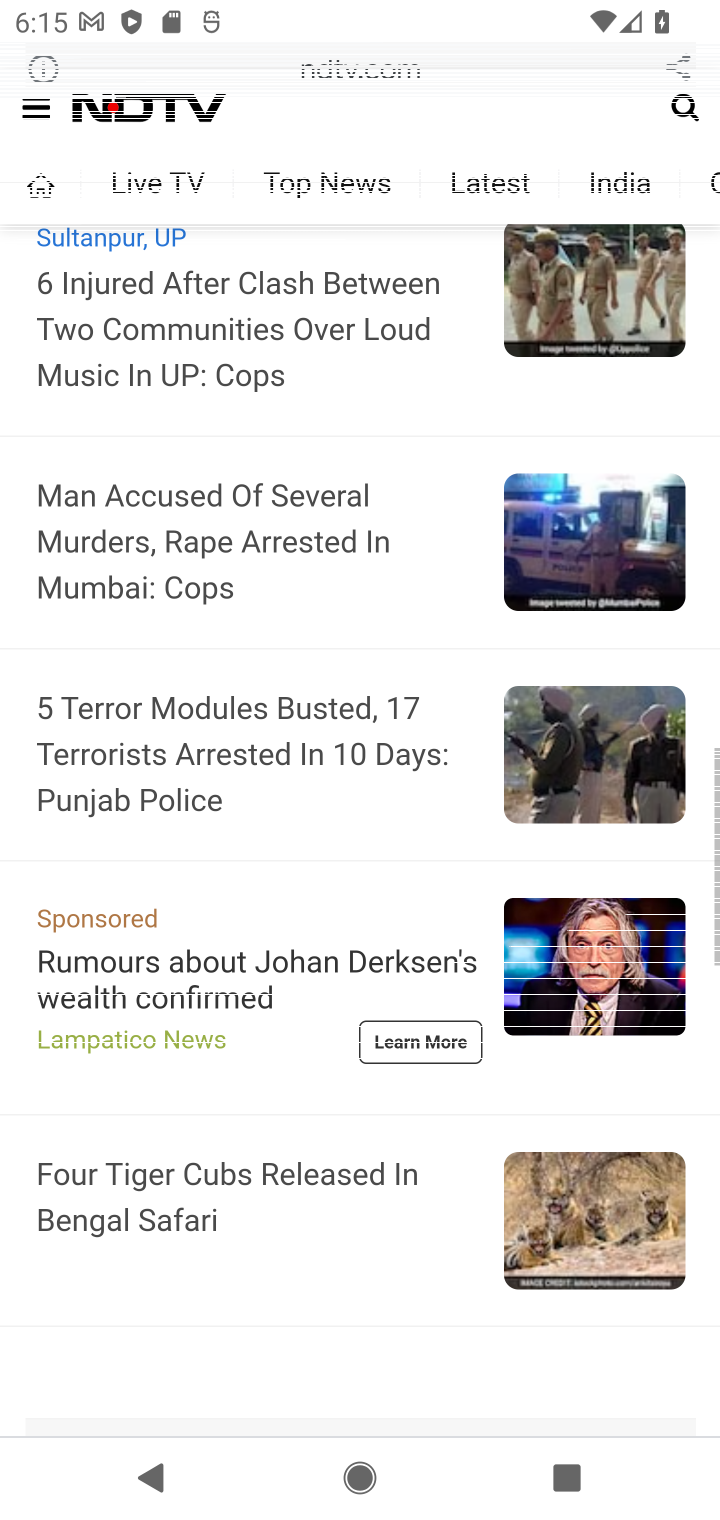
Step 55: click (624, 838)
Your task to perform on an android device: What's the news in India? Image 56: 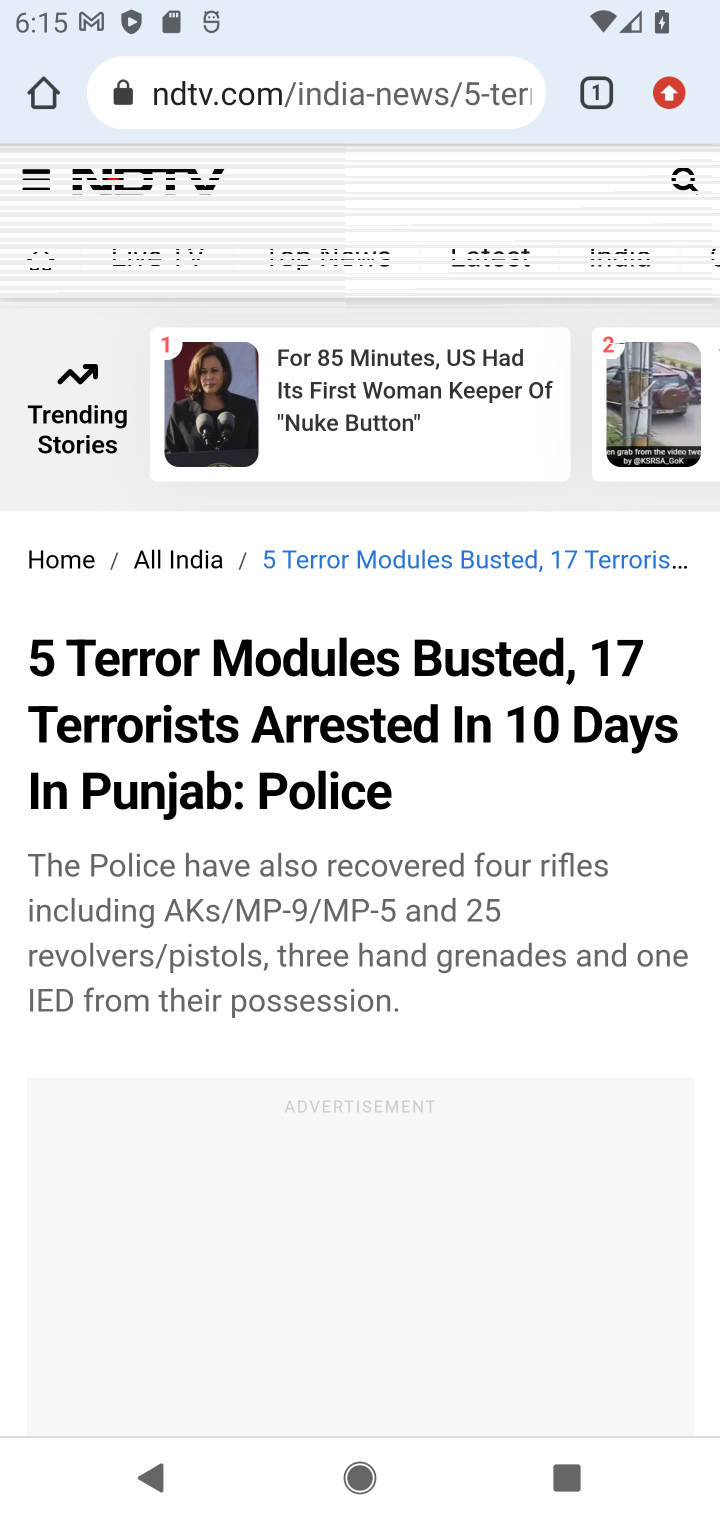
Step 56: drag from (597, 881) to (615, 772)
Your task to perform on an android device: What's the news in India? Image 57: 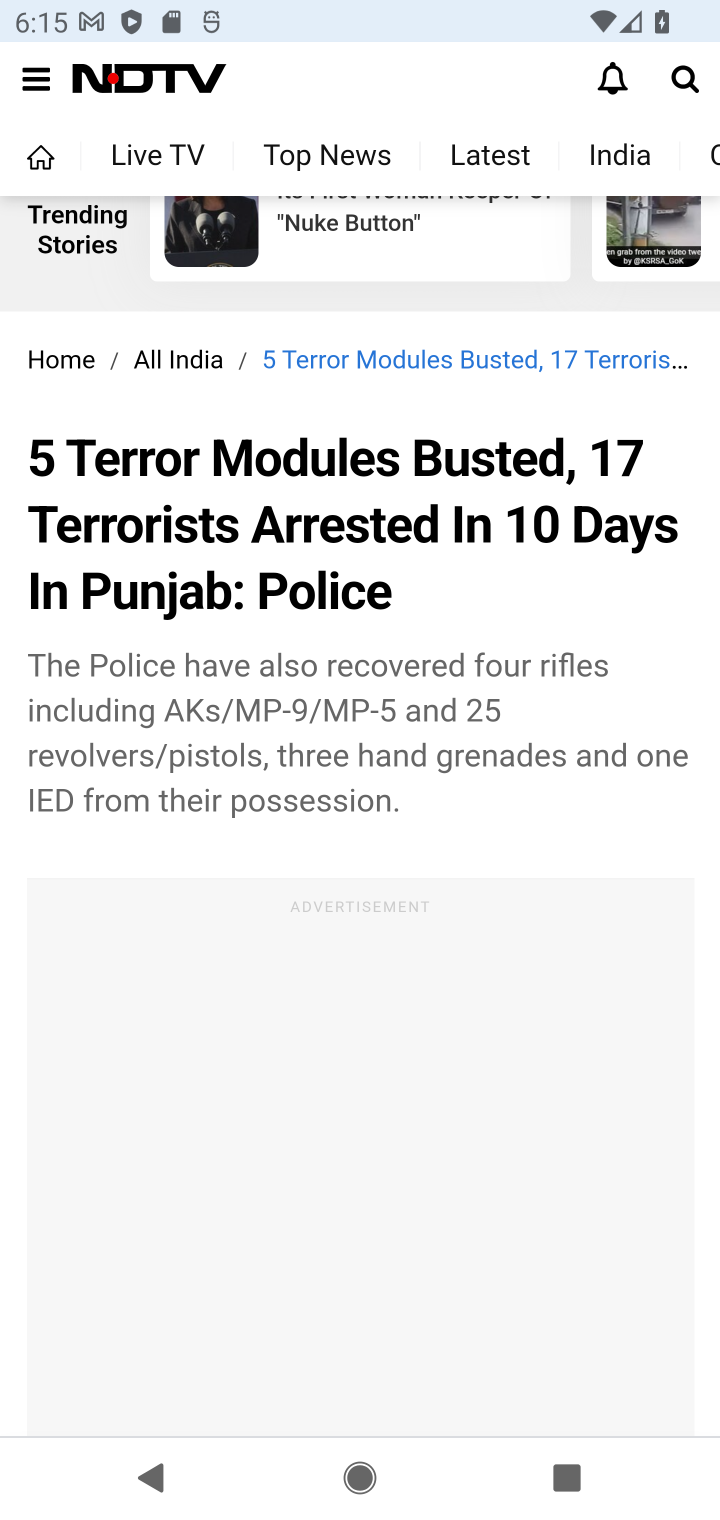
Step 57: drag from (603, 1000) to (579, 668)
Your task to perform on an android device: What's the news in India? Image 58: 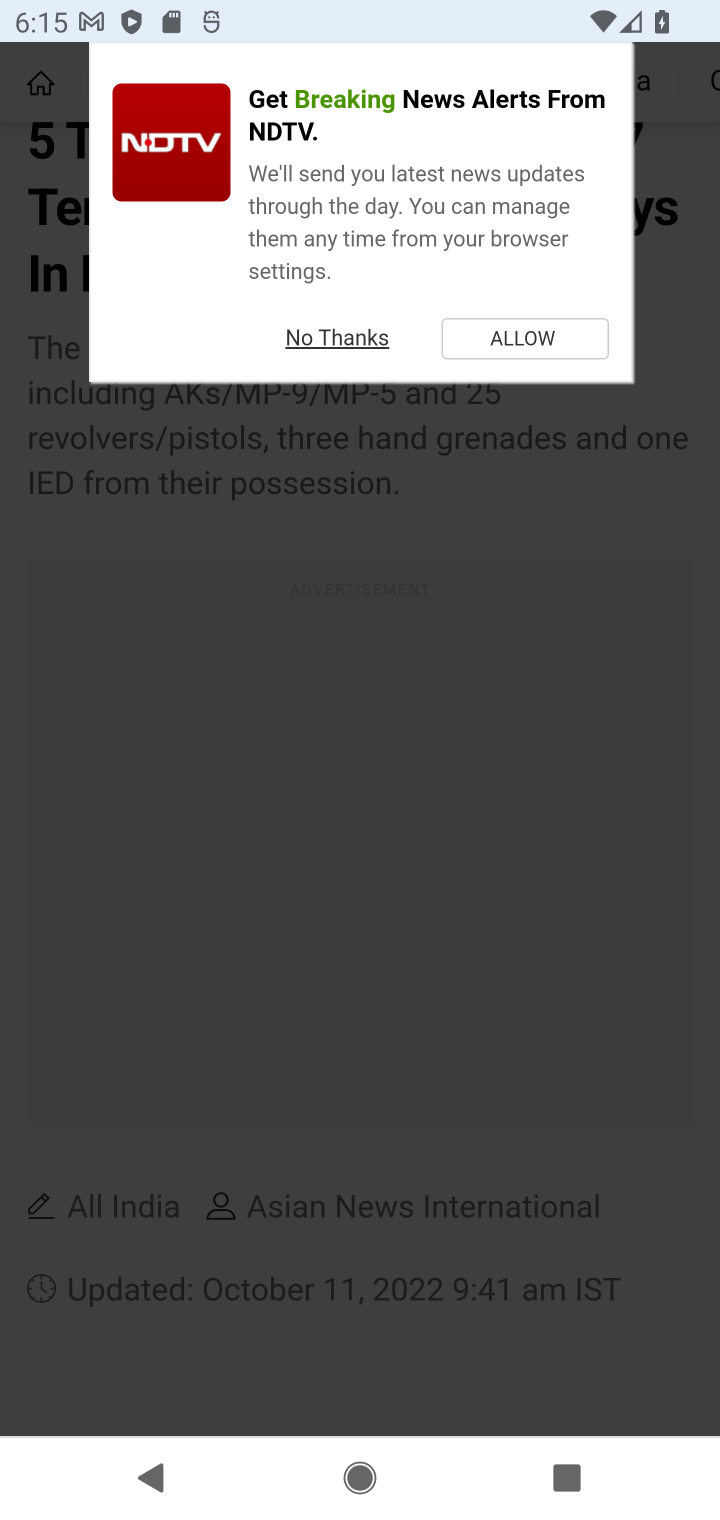
Step 58: click (372, 338)
Your task to perform on an android device: What's the news in India? Image 59: 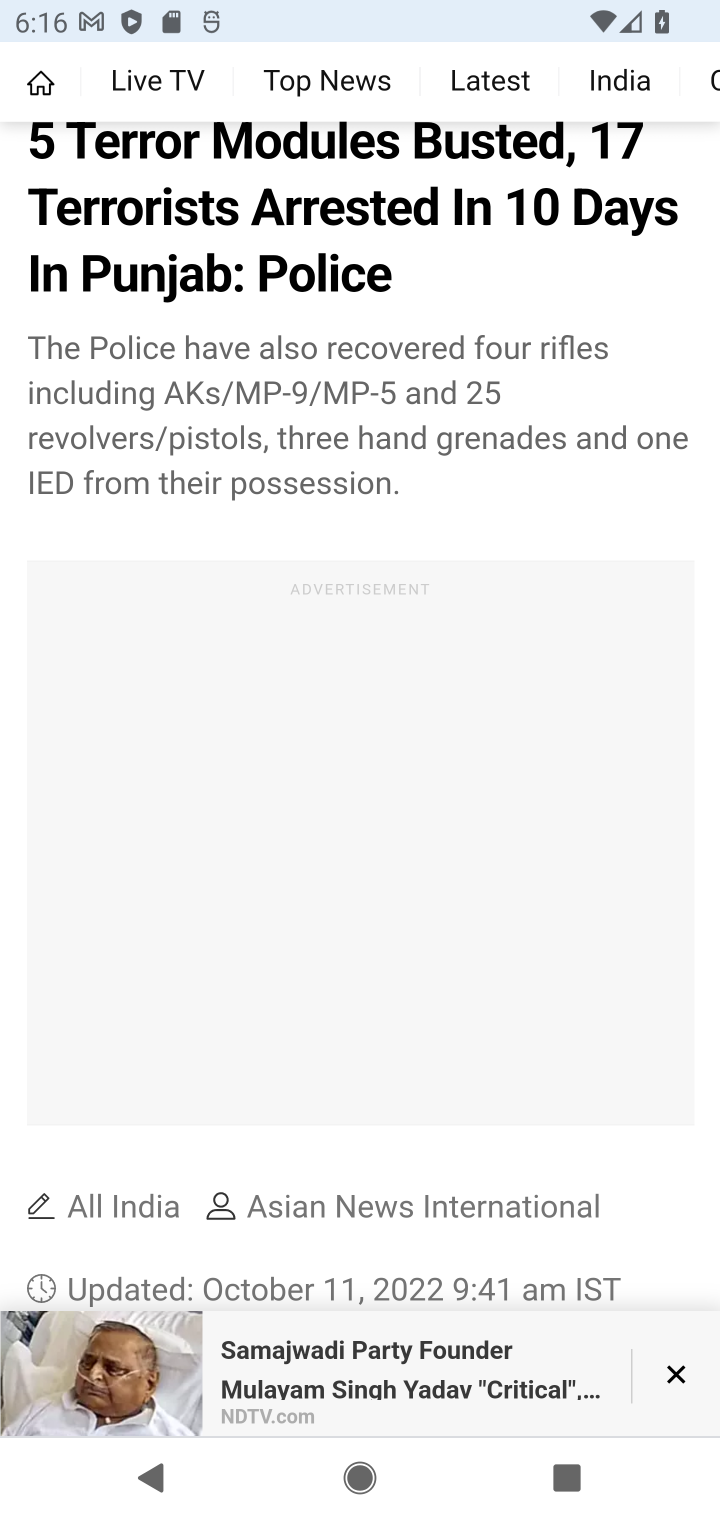
Step 59: click (404, 453)
Your task to perform on an android device: What's the news in India? Image 60: 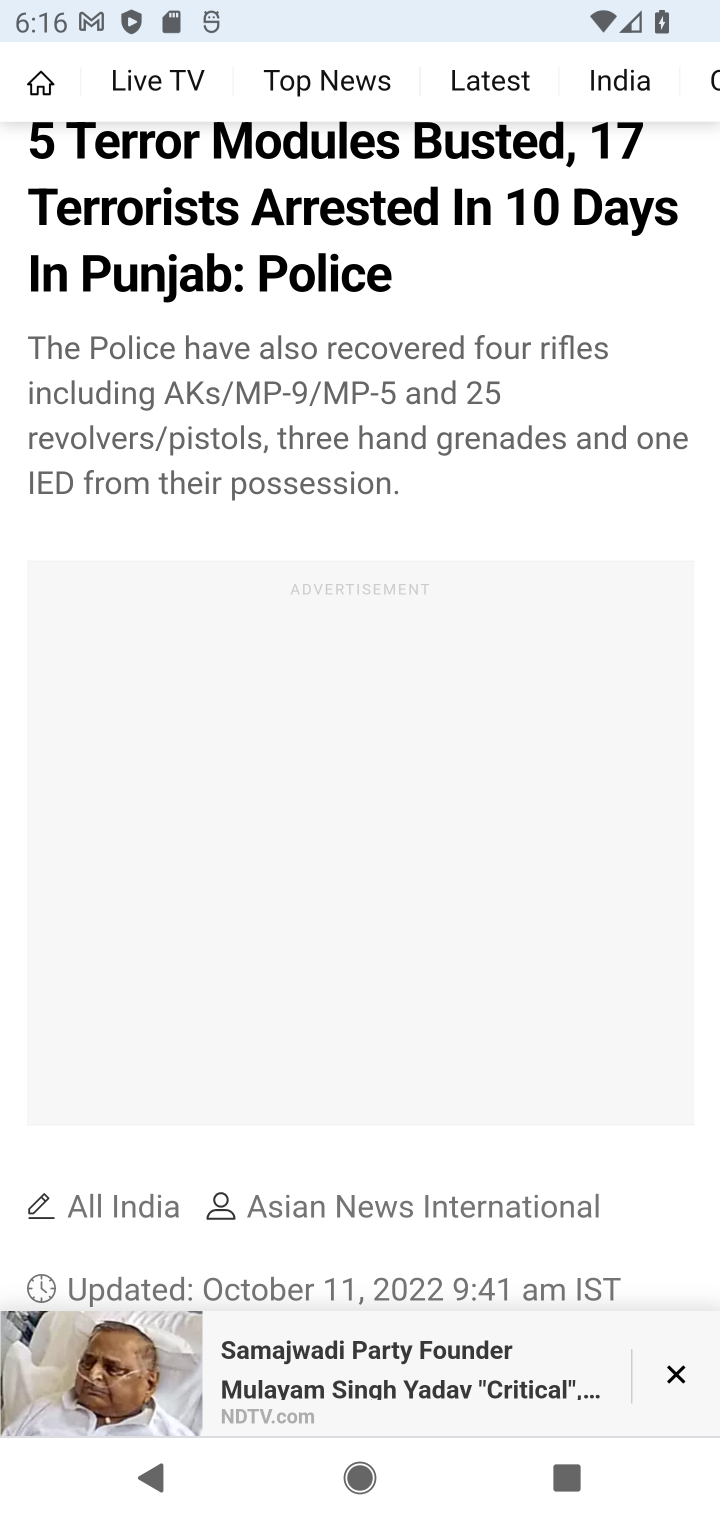
Step 60: drag from (403, 589) to (415, 426)
Your task to perform on an android device: What's the news in India? Image 61: 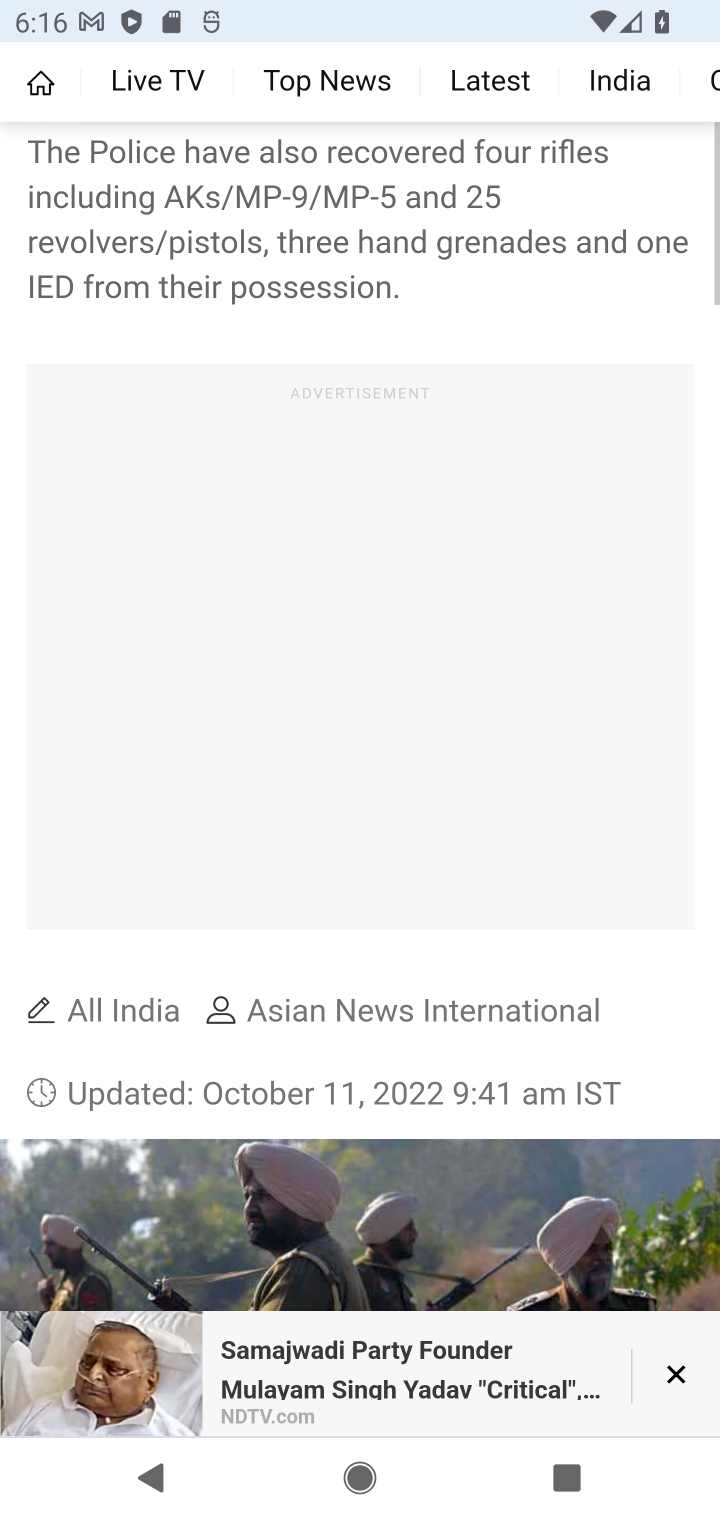
Step 61: drag from (427, 692) to (459, 330)
Your task to perform on an android device: What's the news in India? Image 62: 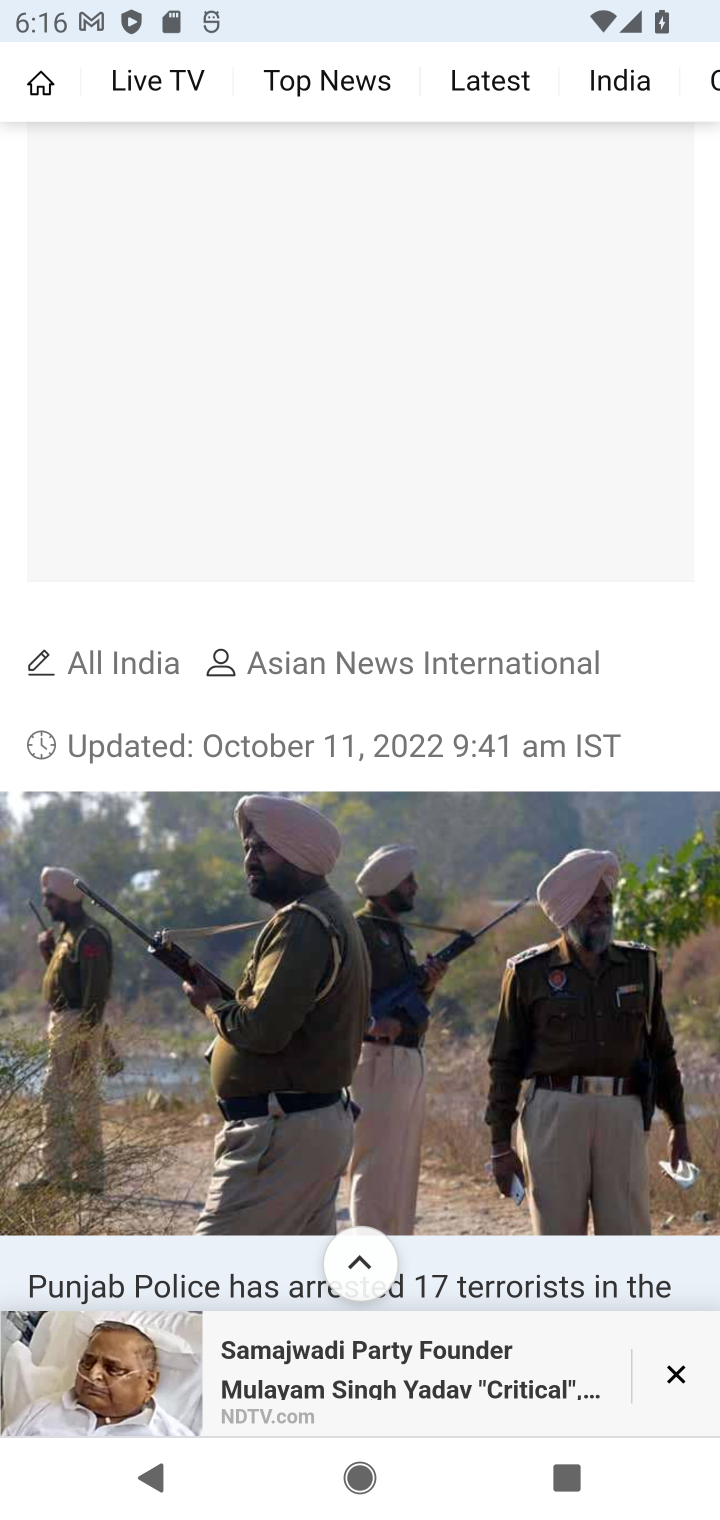
Step 62: drag from (455, 499) to (451, 297)
Your task to perform on an android device: What's the news in India? Image 63: 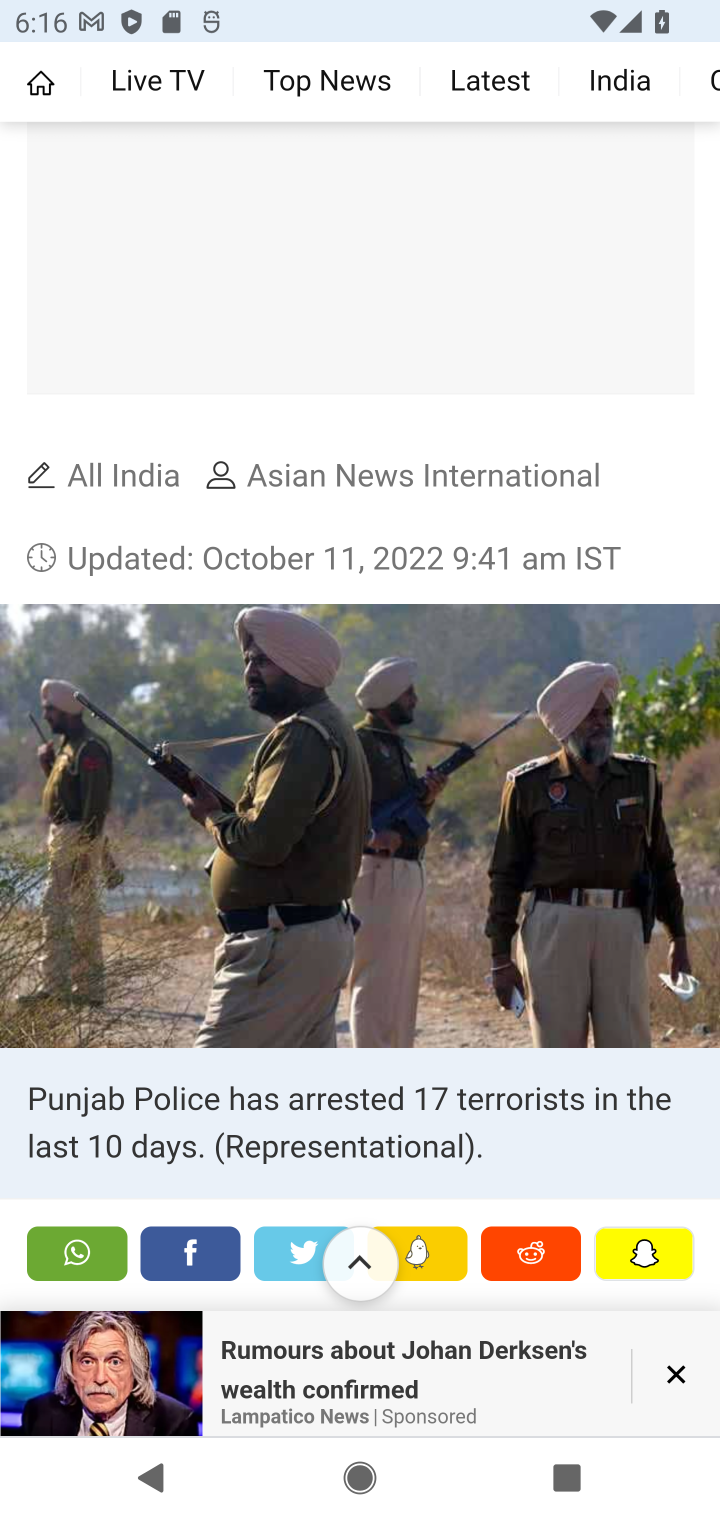
Step 63: drag from (450, 861) to (390, 288)
Your task to perform on an android device: What's the news in India? Image 64: 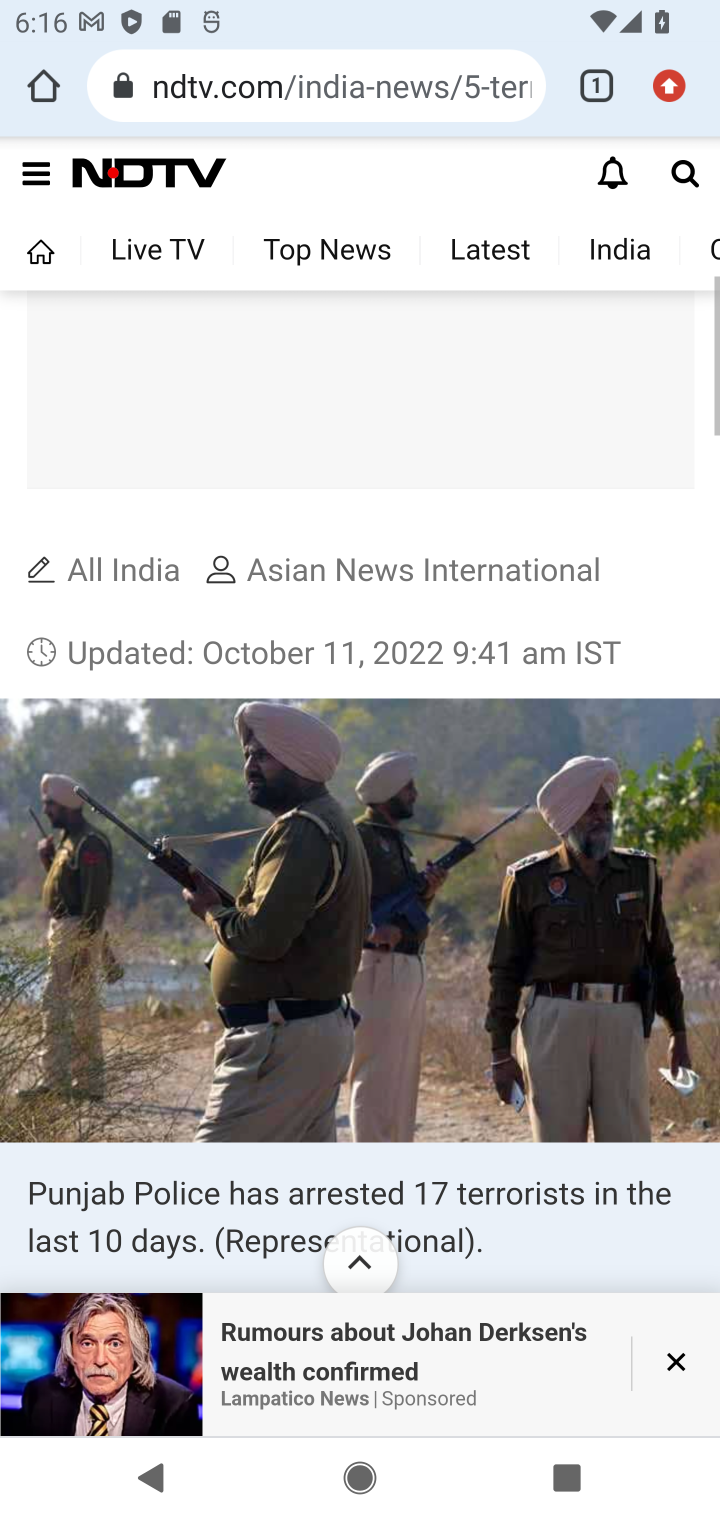
Step 64: click (379, 530)
Your task to perform on an android device: What's the news in India? Image 65: 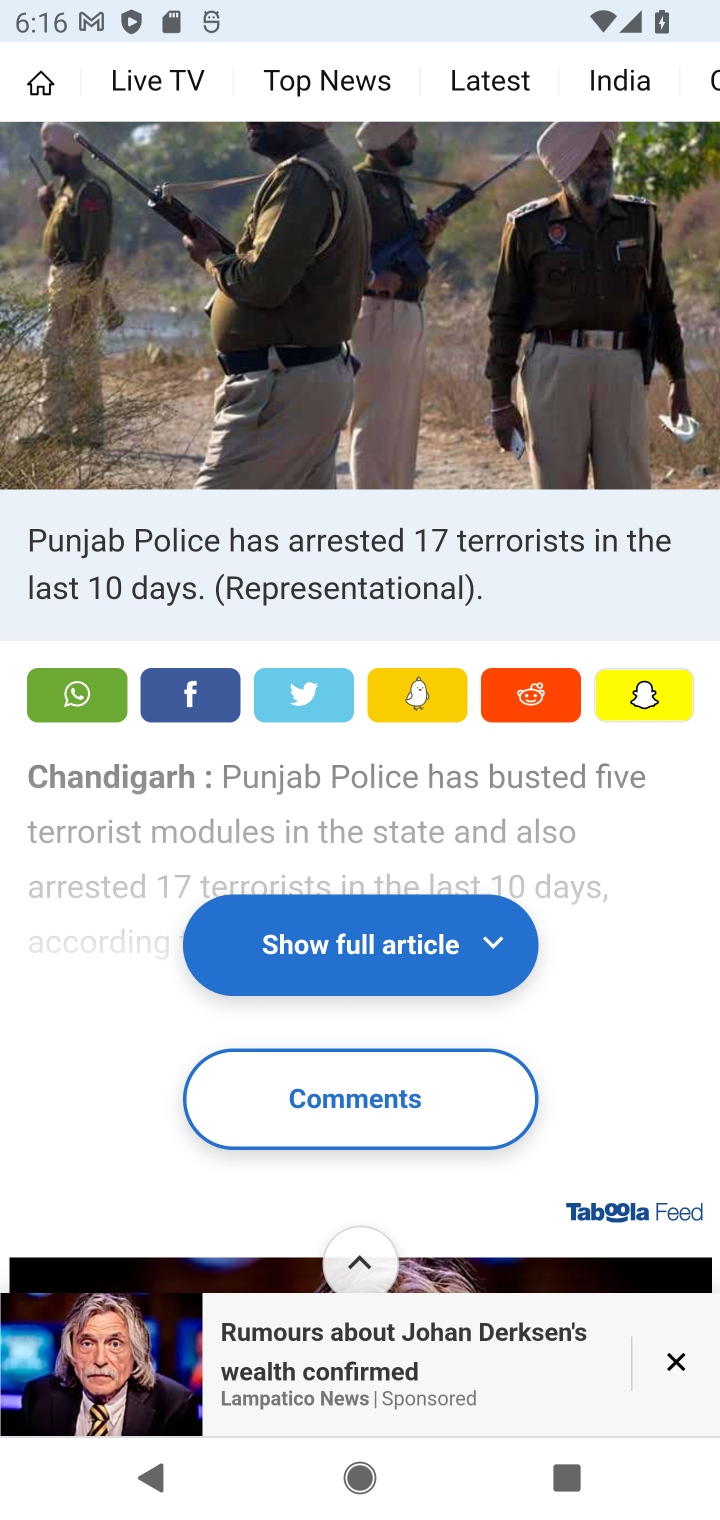
Step 65: task complete